Your task to perform on an android device: Open a new incognito window in Chrome Image 0: 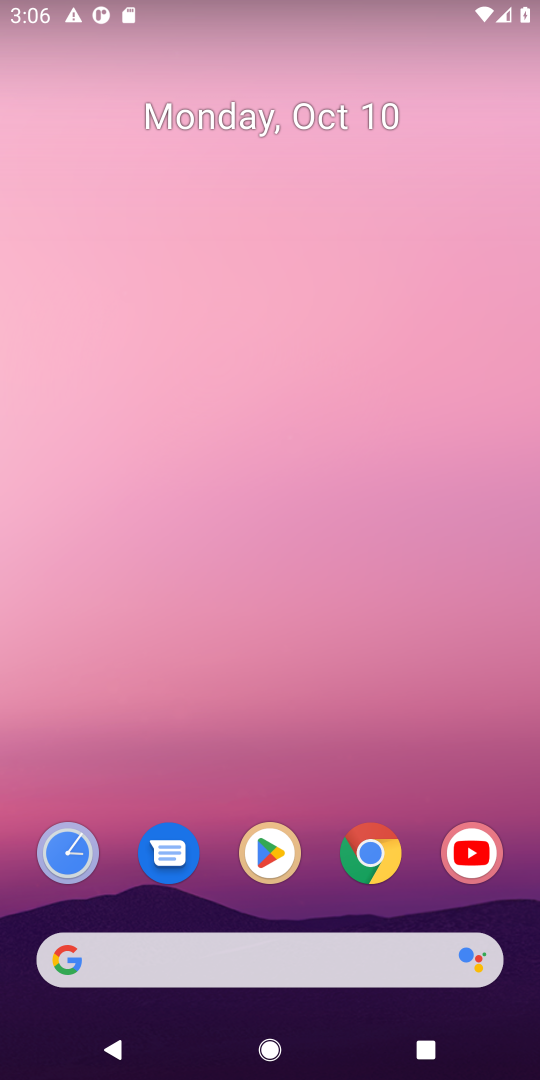
Step 0: click (369, 857)
Your task to perform on an android device: Open a new incognito window in Chrome Image 1: 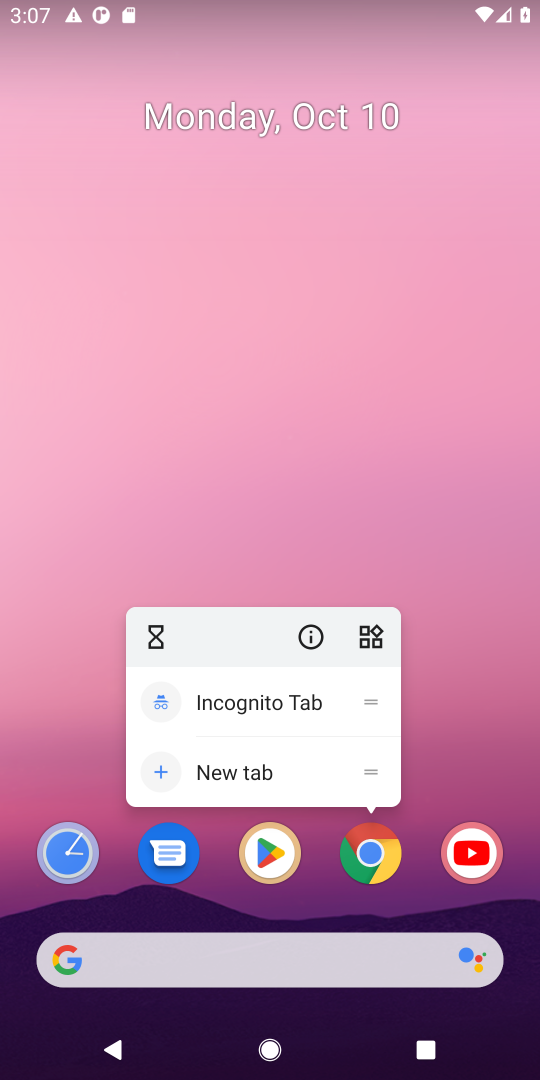
Step 1: click (357, 869)
Your task to perform on an android device: Open a new incognito window in Chrome Image 2: 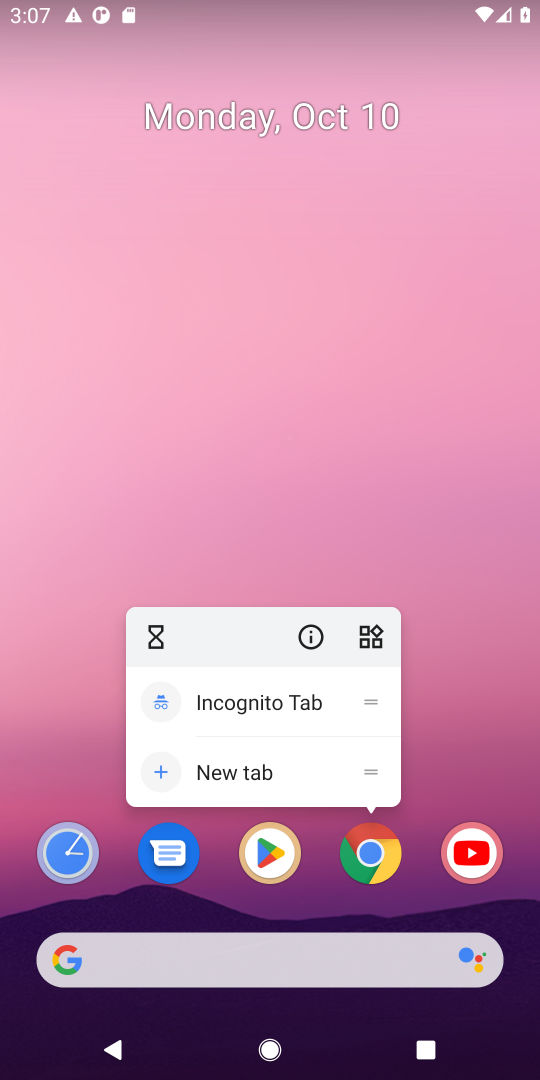
Step 2: click (396, 895)
Your task to perform on an android device: Open a new incognito window in Chrome Image 3: 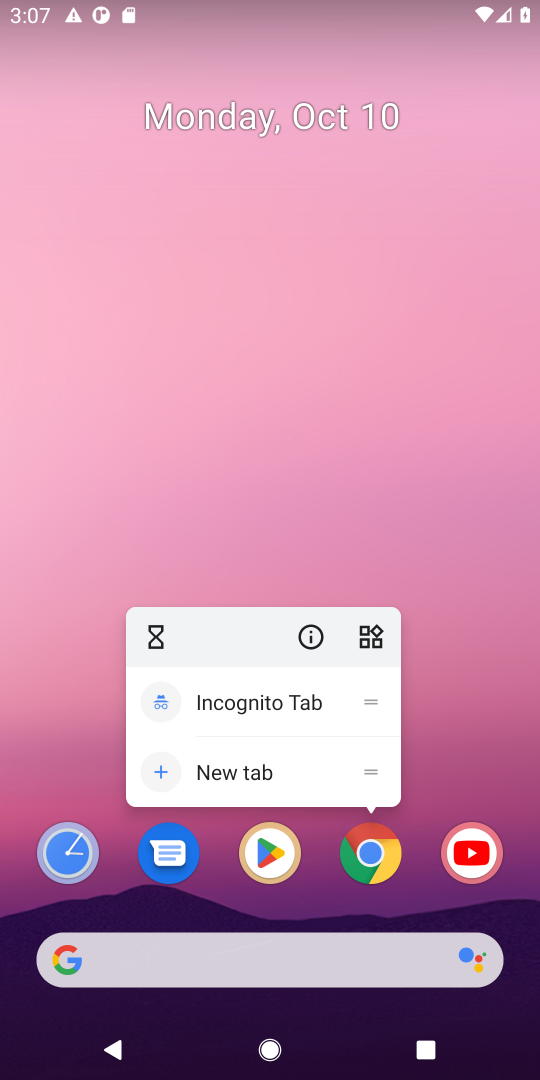
Step 3: click (301, 692)
Your task to perform on an android device: Open a new incognito window in Chrome Image 4: 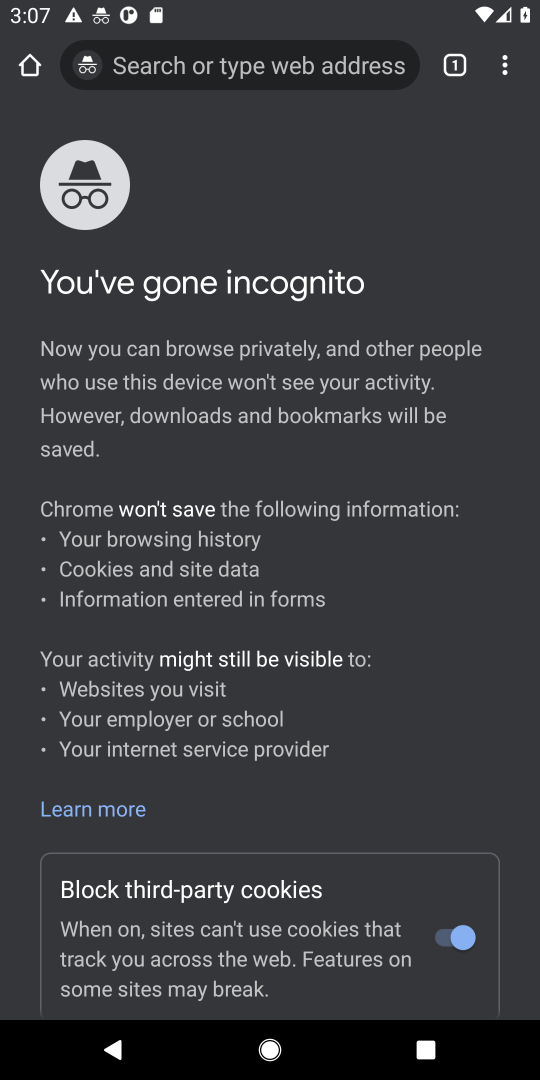
Step 4: drag from (432, 733) to (498, 186)
Your task to perform on an android device: Open a new incognito window in Chrome Image 5: 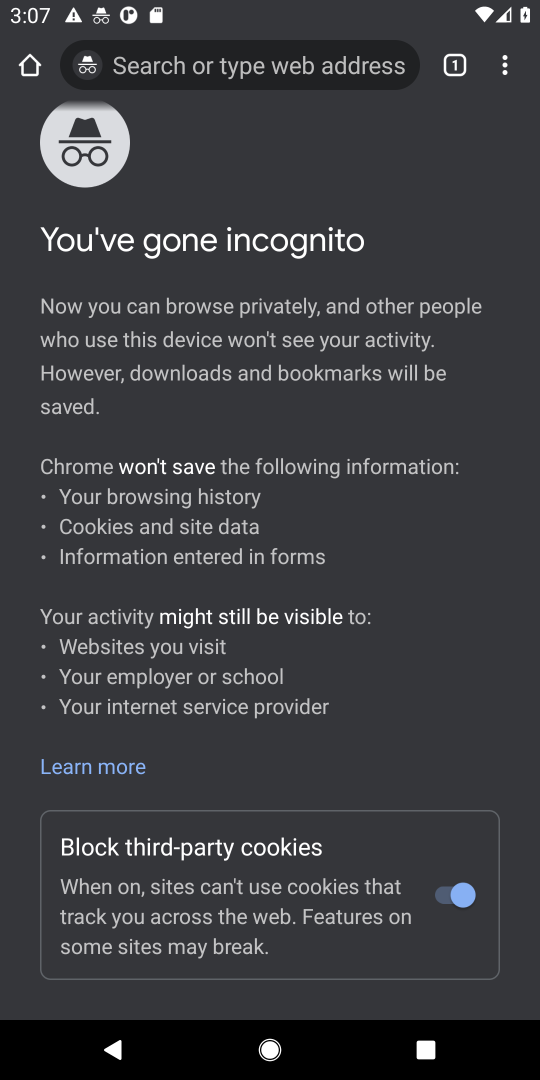
Step 5: drag from (441, 880) to (494, 305)
Your task to perform on an android device: Open a new incognito window in Chrome Image 6: 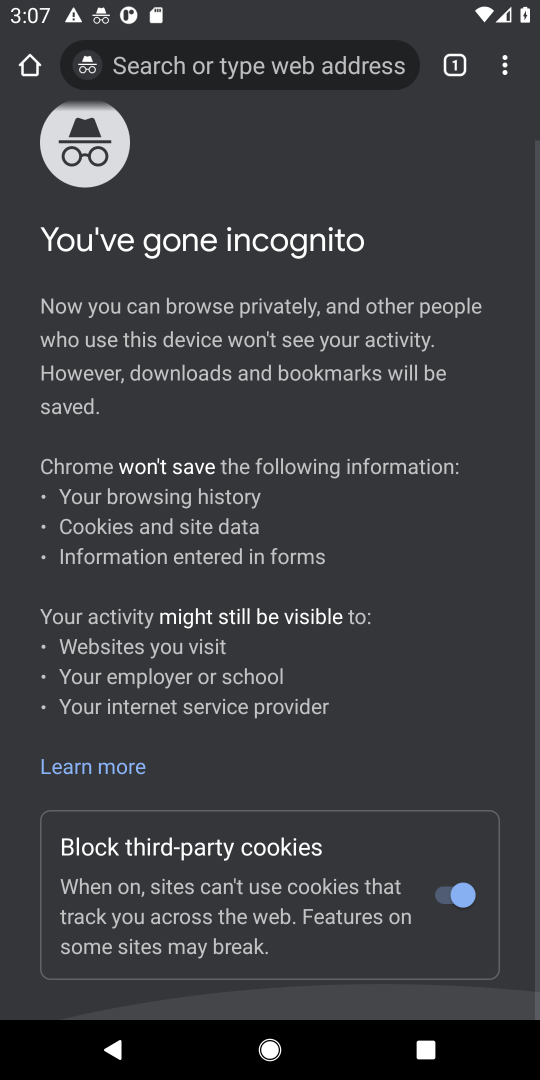
Step 6: click (131, 766)
Your task to perform on an android device: Open a new incognito window in Chrome Image 7: 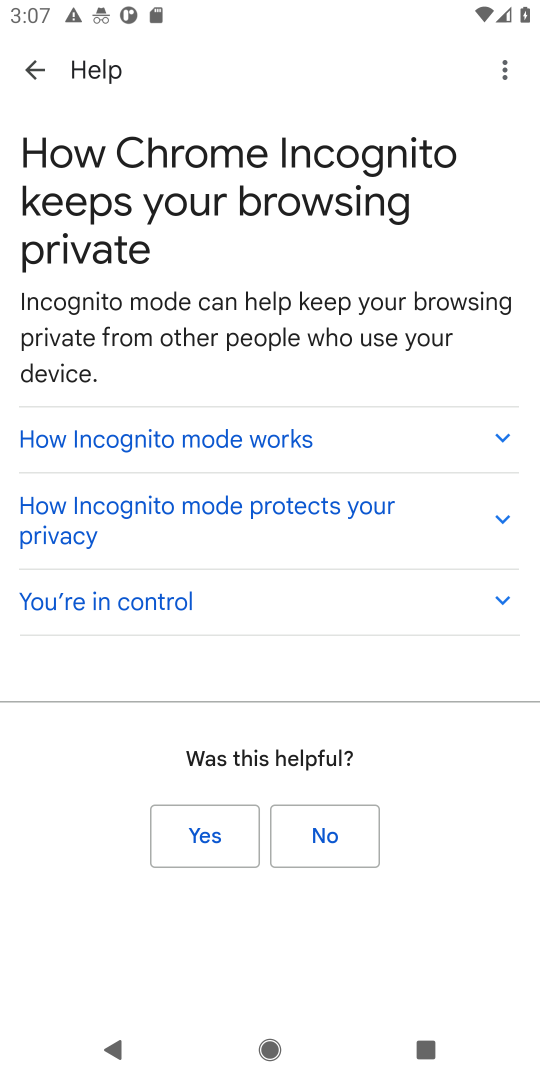
Step 7: click (348, 856)
Your task to perform on an android device: Open a new incognito window in Chrome Image 8: 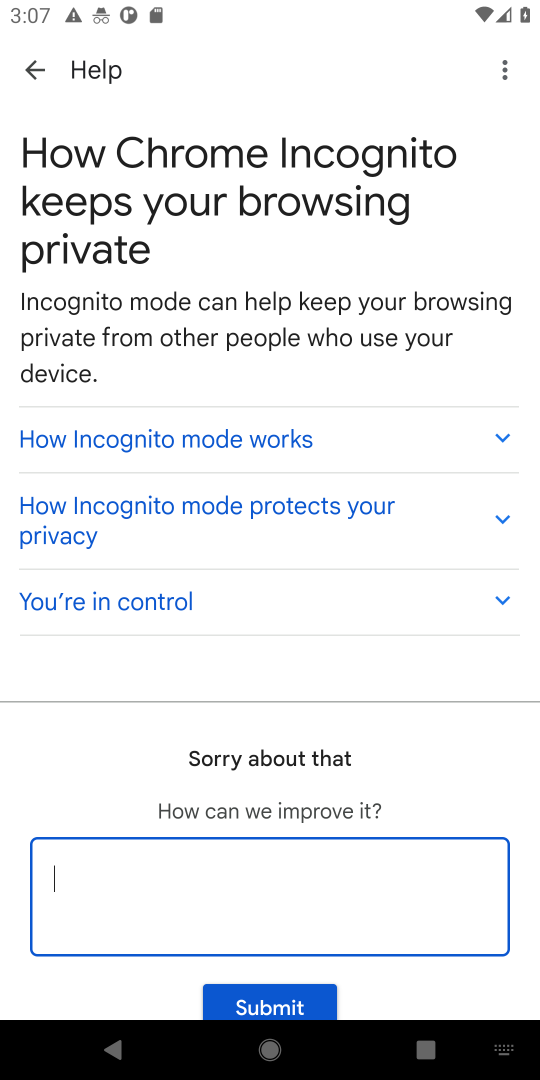
Step 8: drag from (373, 745) to (370, 140)
Your task to perform on an android device: Open a new incognito window in Chrome Image 9: 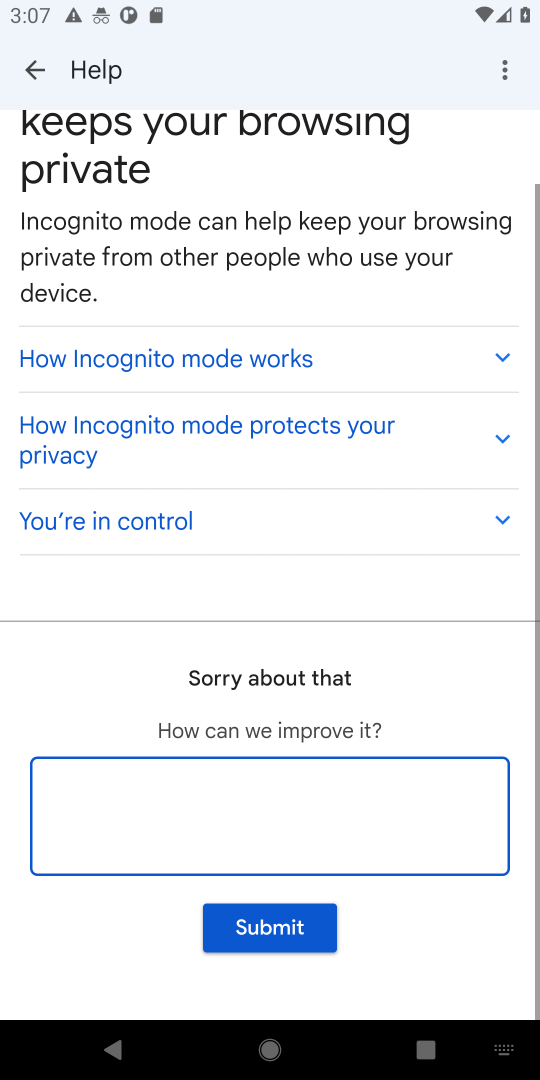
Step 9: click (28, 72)
Your task to perform on an android device: Open a new incognito window in Chrome Image 10: 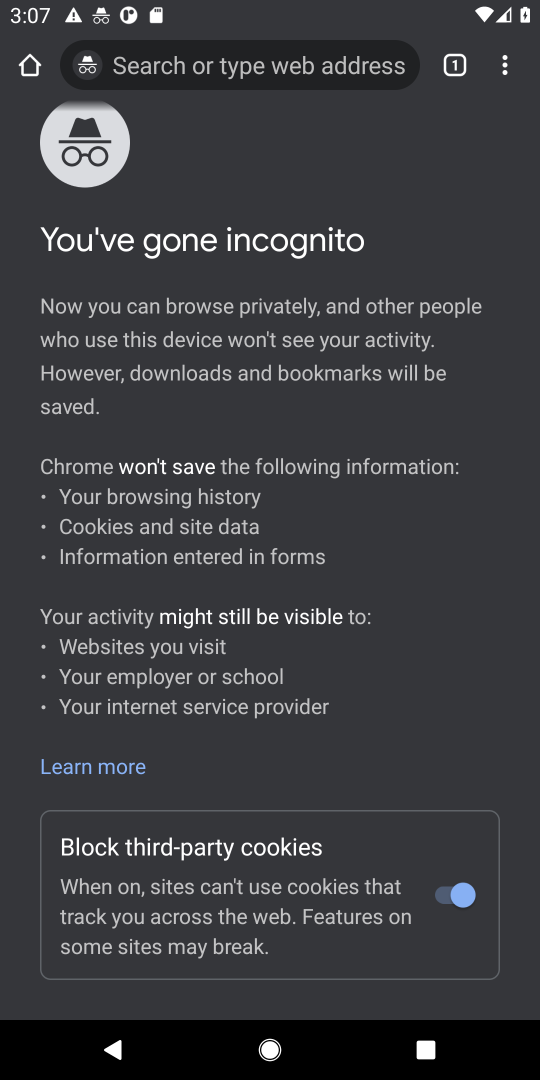
Step 10: drag from (313, 357) to (334, 130)
Your task to perform on an android device: Open a new incognito window in Chrome Image 11: 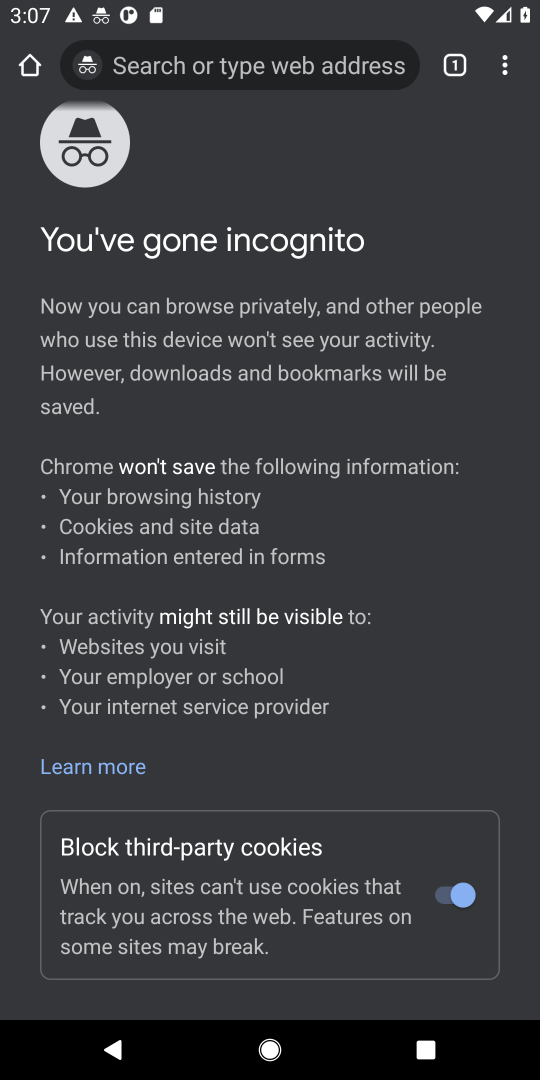
Step 11: drag from (375, 392) to (384, 241)
Your task to perform on an android device: Open a new incognito window in Chrome Image 12: 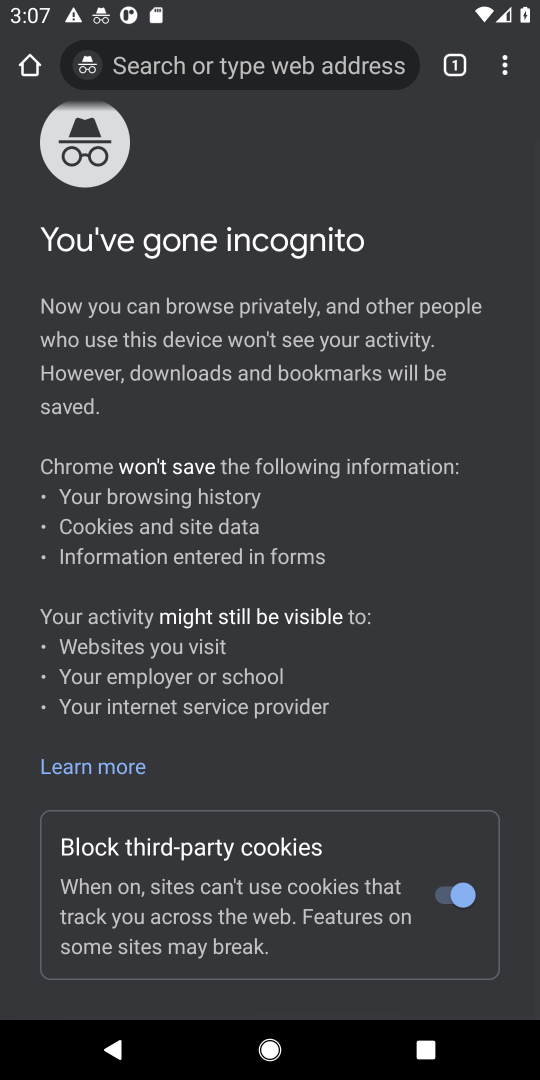
Step 12: click (212, 70)
Your task to perform on an android device: Open a new incognito window in Chrome Image 13: 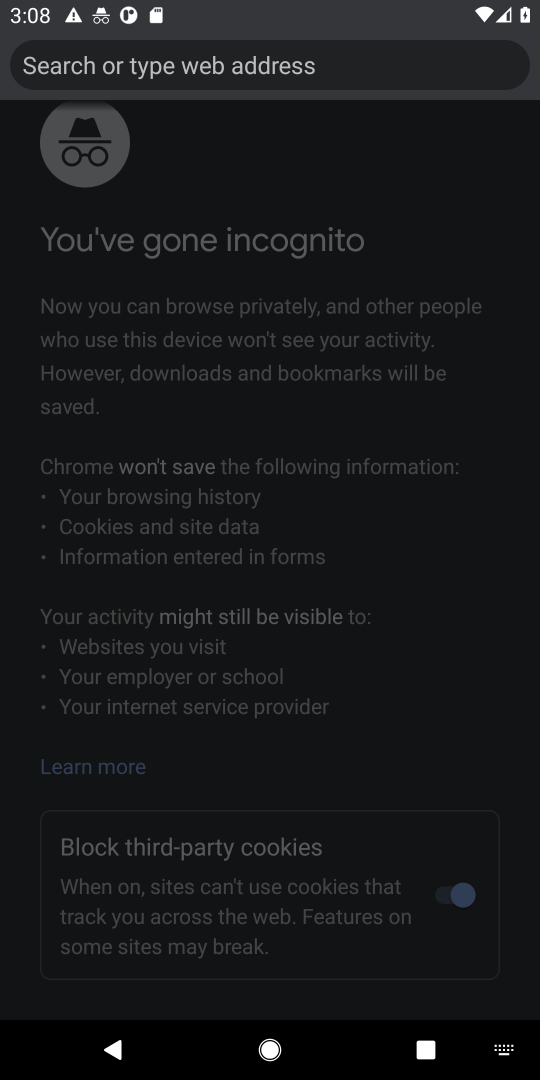
Step 13: type "cars"
Your task to perform on an android device: Open a new incognito window in Chrome Image 14: 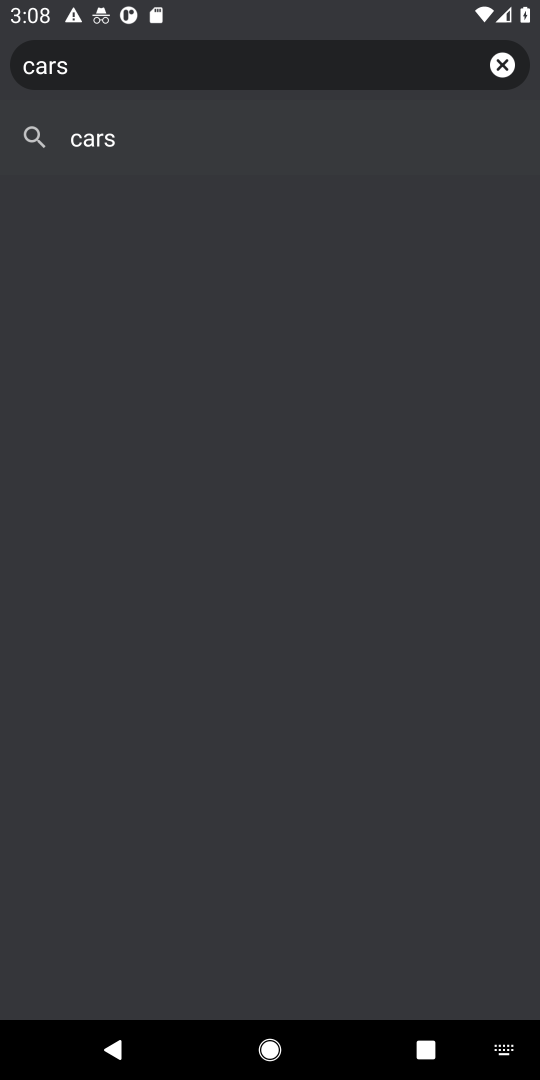
Step 14: press enter
Your task to perform on an android device: Open a new incognito window in Chrome Image 15: 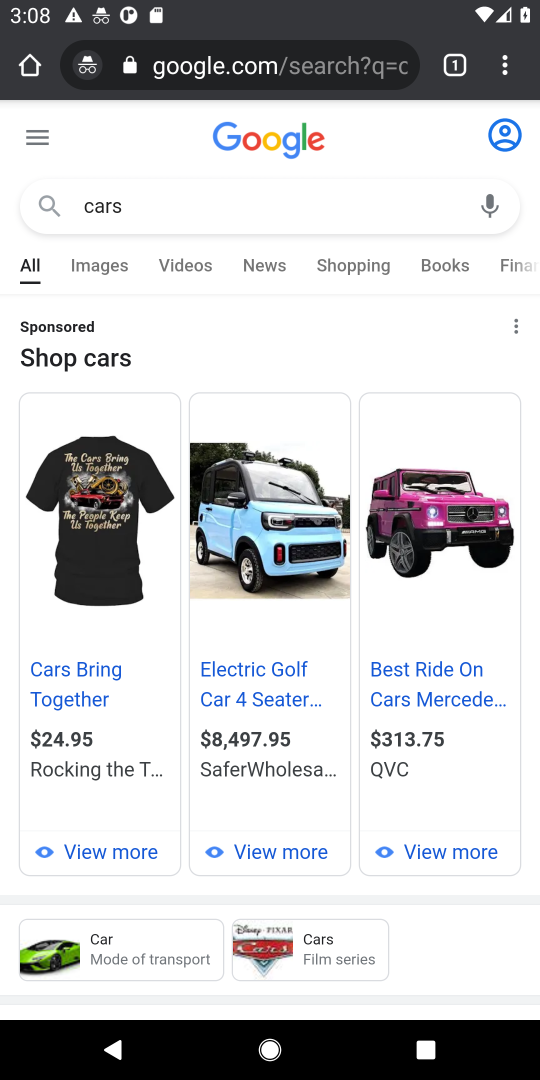
Step 15: drag from (424, 862) to (396, 96)
Your task to perform on an android device: Open a new incognito window in Chrome Image 16: 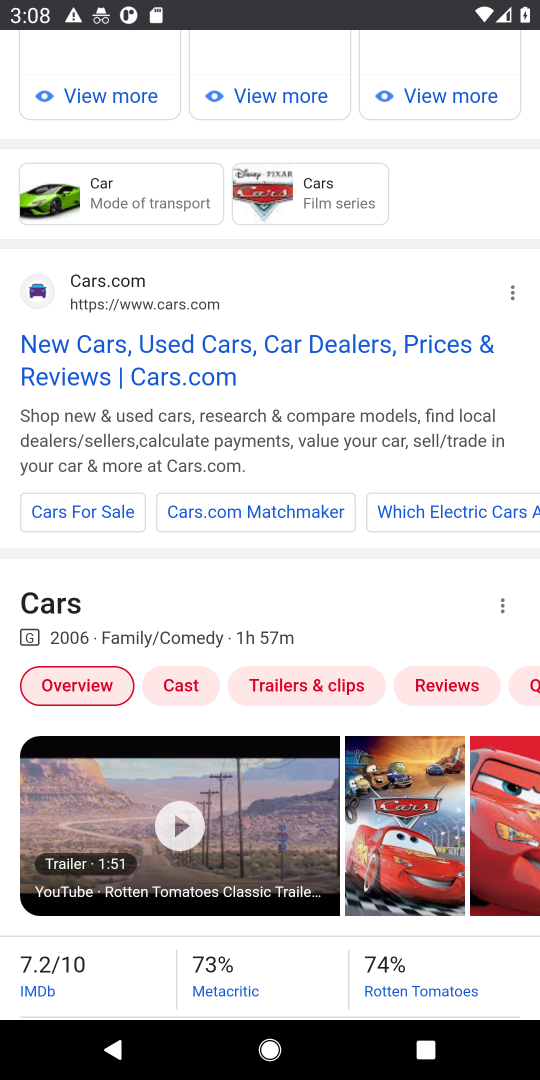
Step 16: click (242, 343)
Your task to perform on an android device: Open a new incognito window in Chrome Image 17: 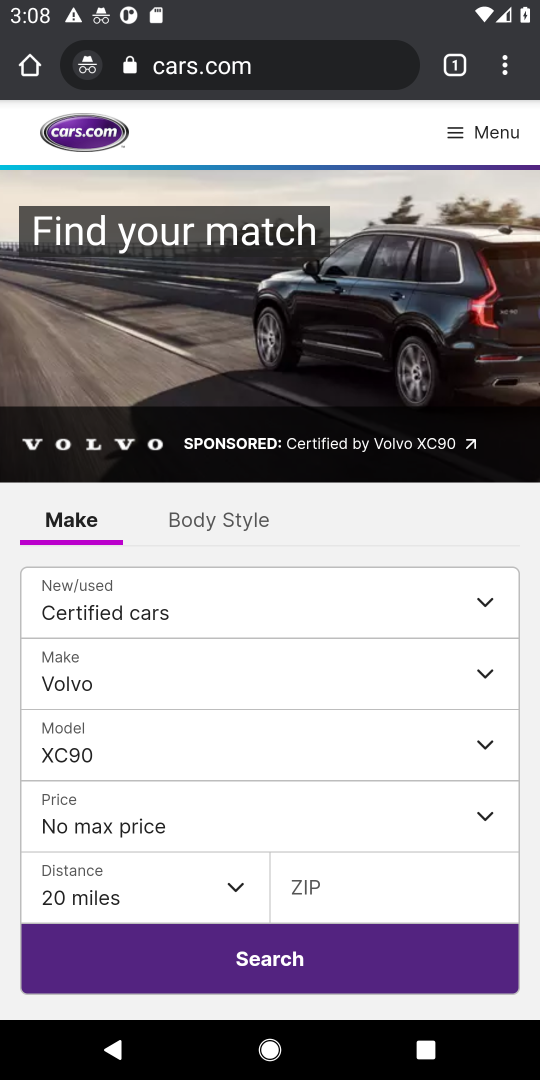
Step 17: drag from (270, 580) to (402, 117)
Your task to perform on an android device: Open a new incognito window in Chrome Image 18: 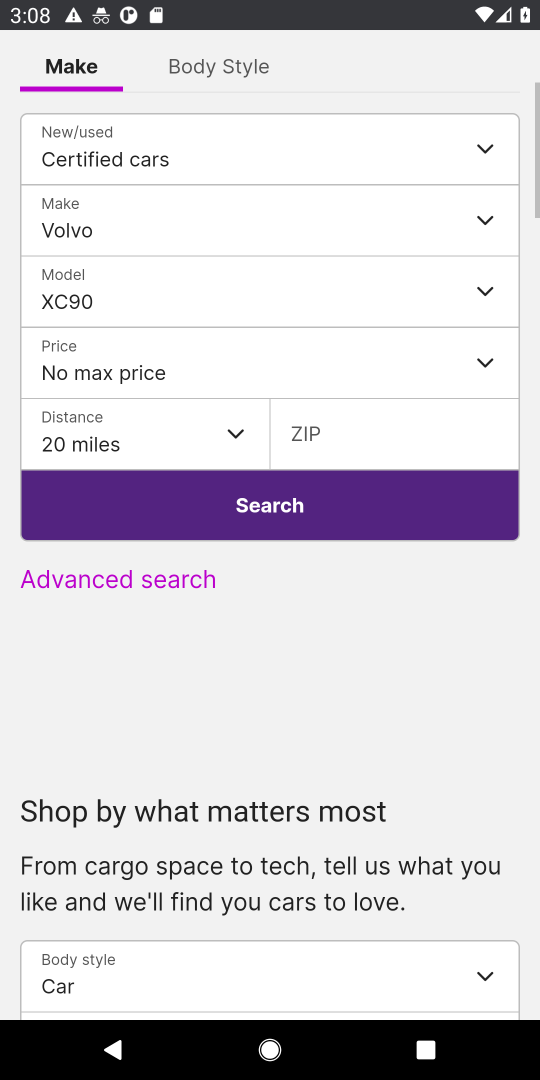
Step 18: drag from (445, 410) to (498, 110)
Your task to perform on an android device: Open a new incognito window in Chrome Image 19: 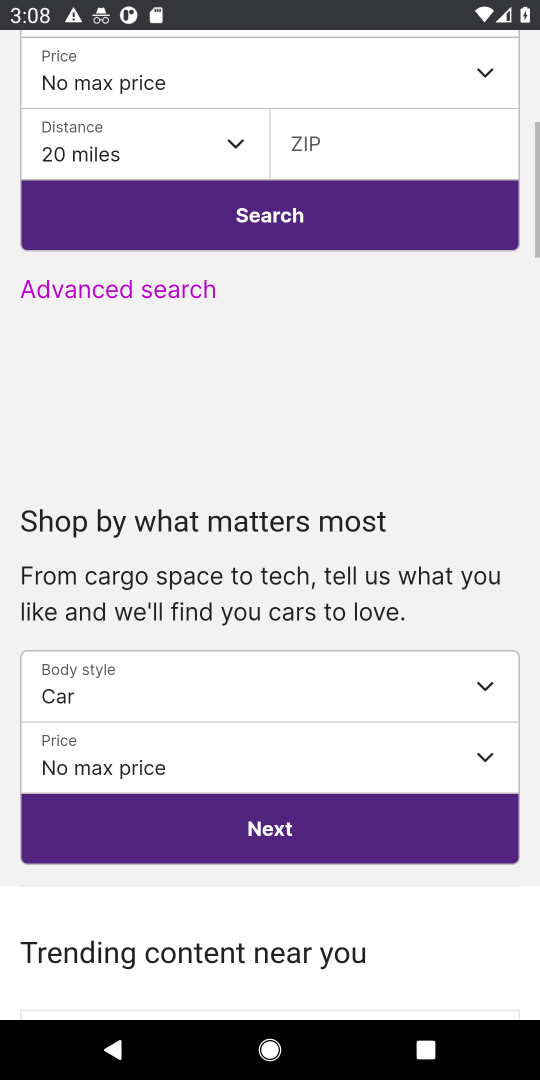
Step 19: drag from (390, 605) to (470, 225)
Your task to perform on an android device: Open a new incognito window in Chrome Image 20: 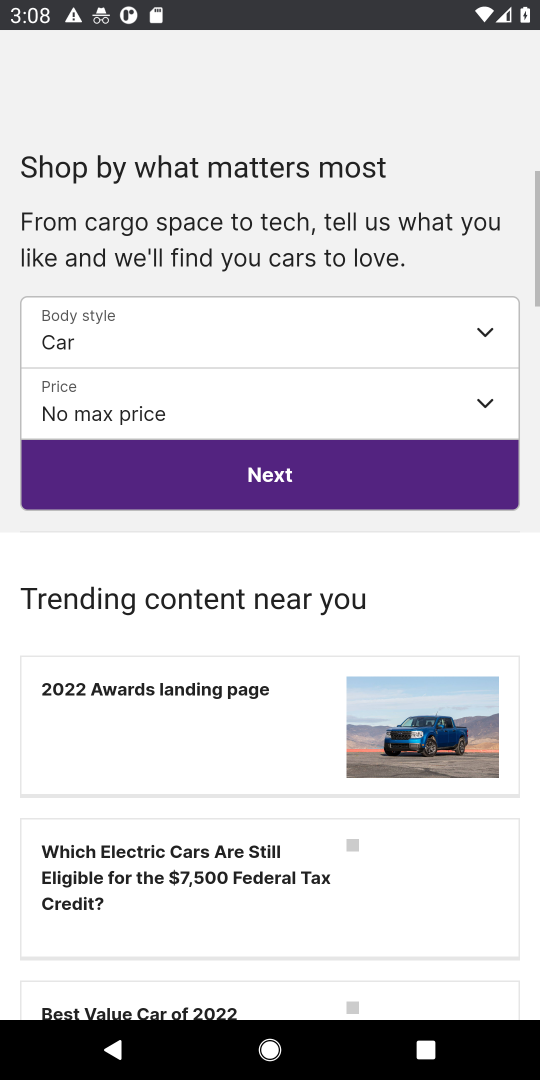
Step 20: drag from (420, 657) to (469, 151)
Your task to perform on an android device: Open a new incognito window in Chrome Image 21: 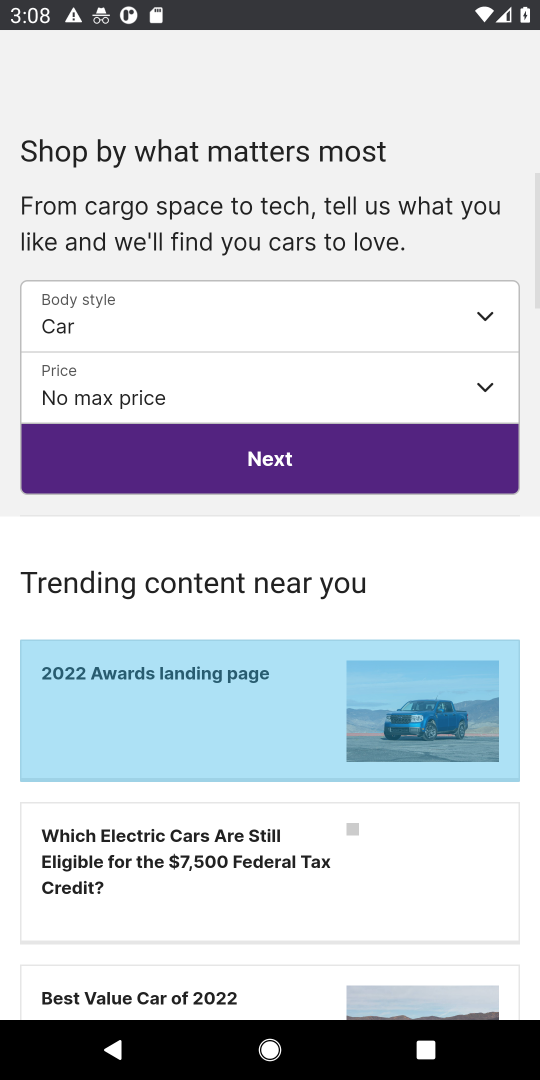
Step 21: drag from (410, 689) to (286, 243)
Your task to perform on an android device: Open a new incognito window in Chrome Image 22: 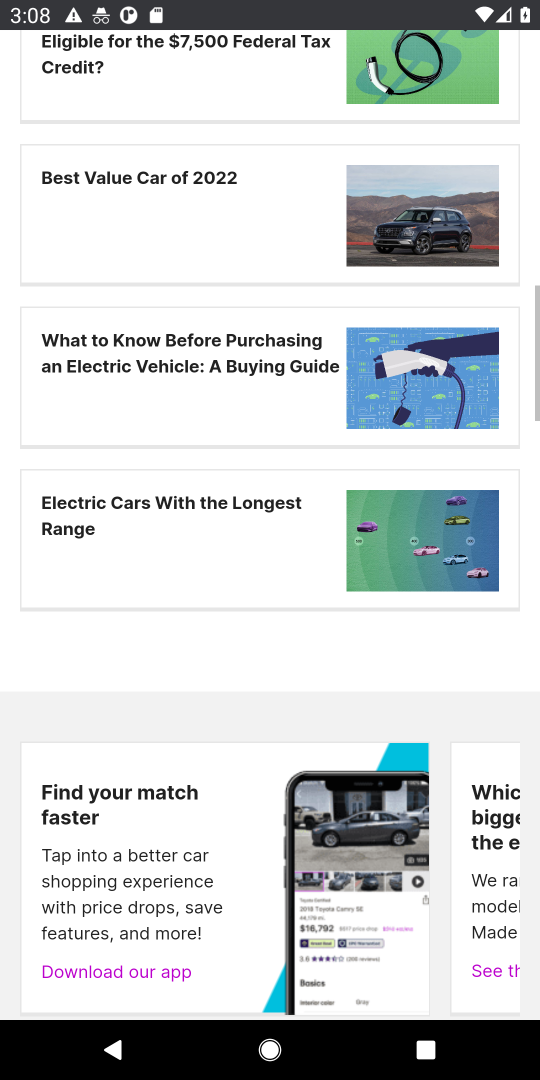
Step 22: drag from (252, 458) to (283, 200)
Your task to perform on an android device: Open a new incognito window in Chrome Image 23: 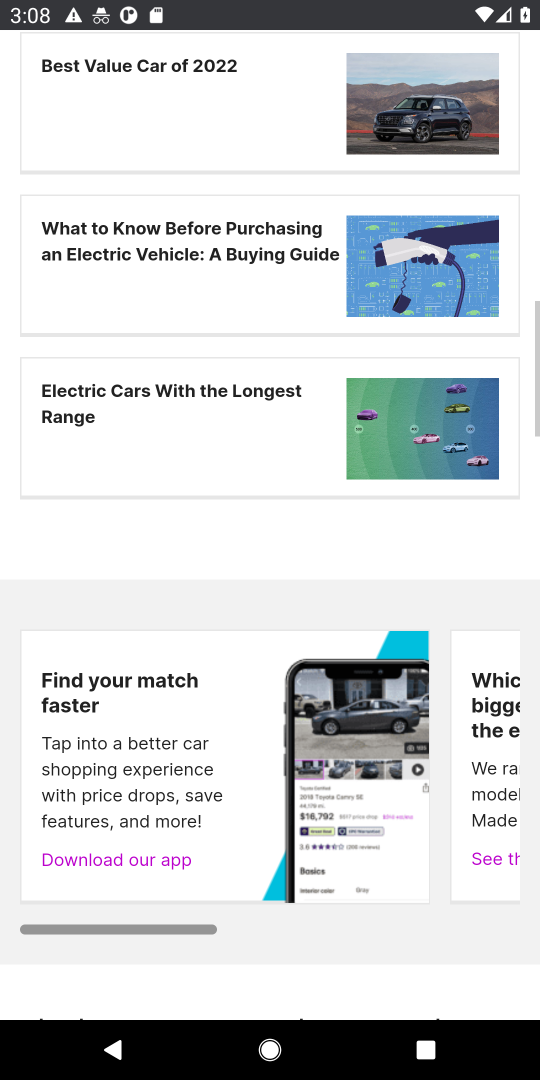
Step 23: drag from (308, 470) to (356, 265)
Your task to perform on an android device: Open a new incognito window in Chrome Image 24: 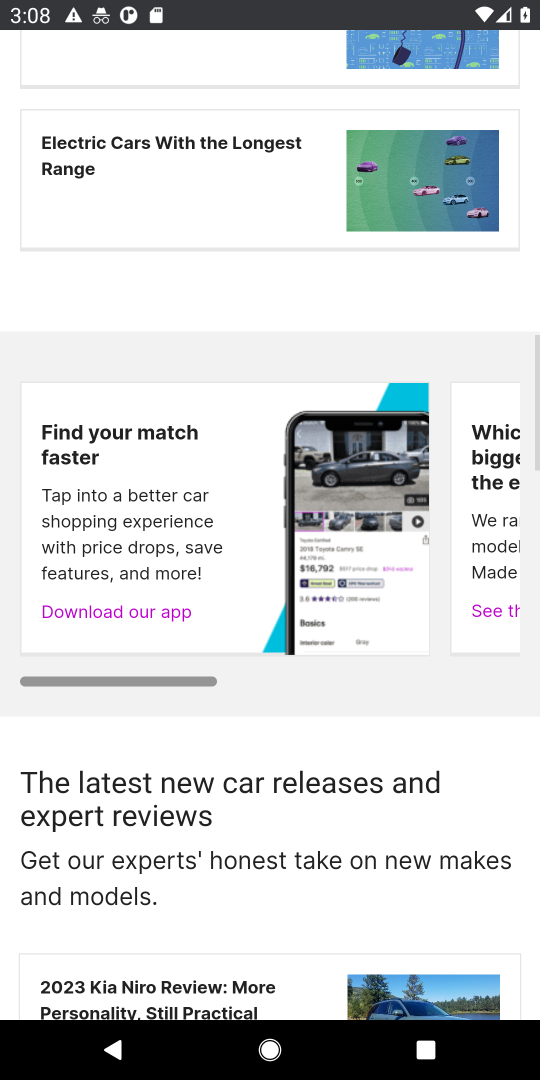
Step 24: drag from (307, 668) to (357, 192)
Your task to perform on an android device: Open a new incognito window in Chrome Image 25: 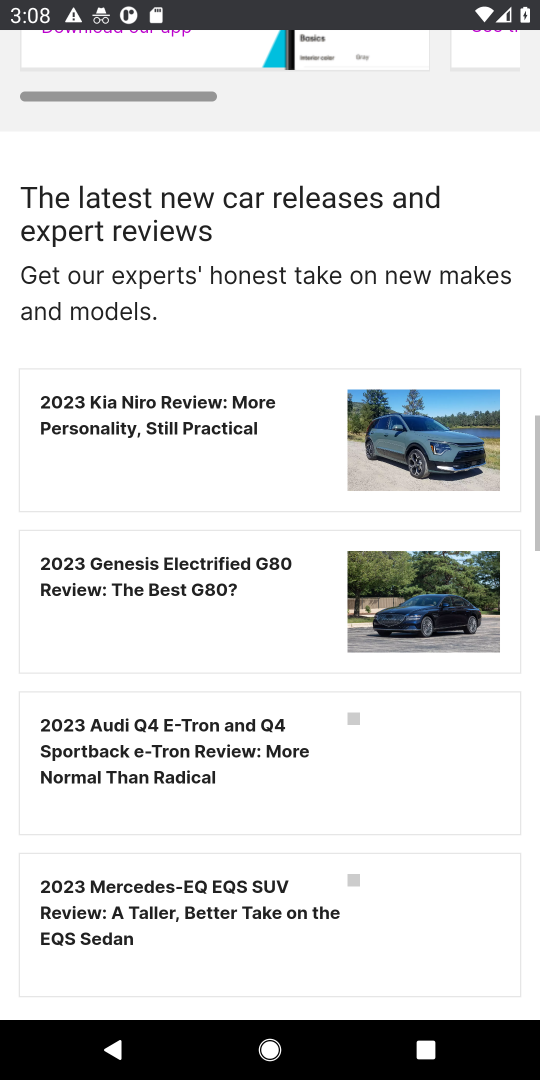
Step 25: drag from (375, 337) to (385, 184)
Your task to perform on an android device: Open a new incognito window in Chrome Image 26: 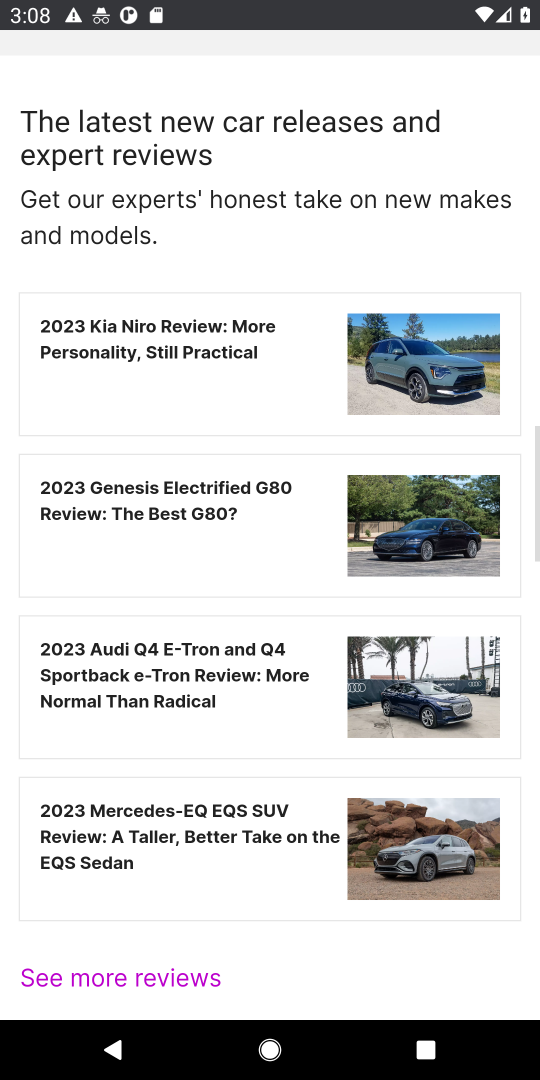
Step 26: drag from (324, 525) to (381, 121)
Your task to perform on an android device: Open a new incognito window in Chrome Image 27: 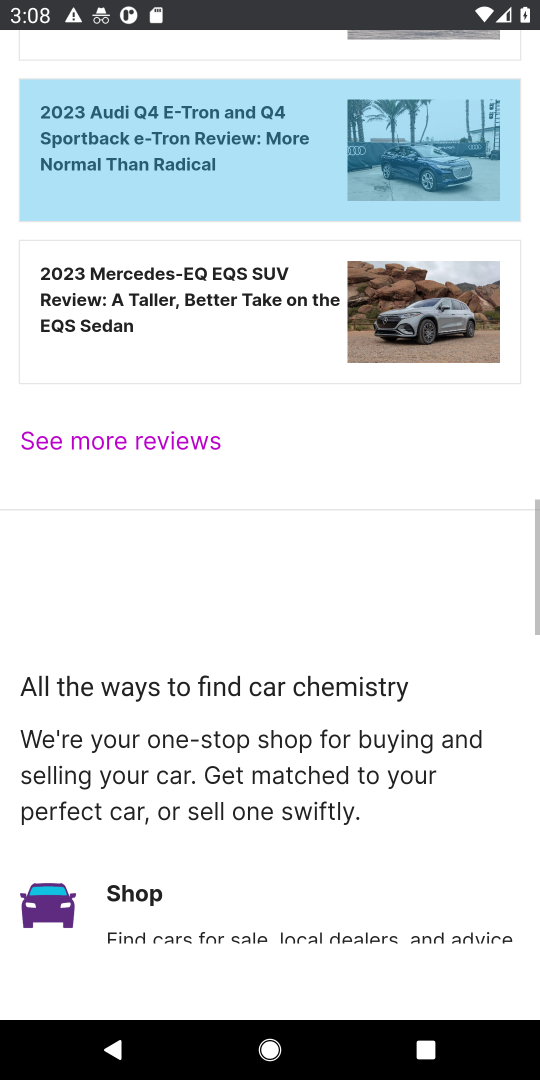
Step 27: drag from (281, 705) to (334, 93)
Your task to perform on an android device: Open a new incognito window in Chrome Image 28: 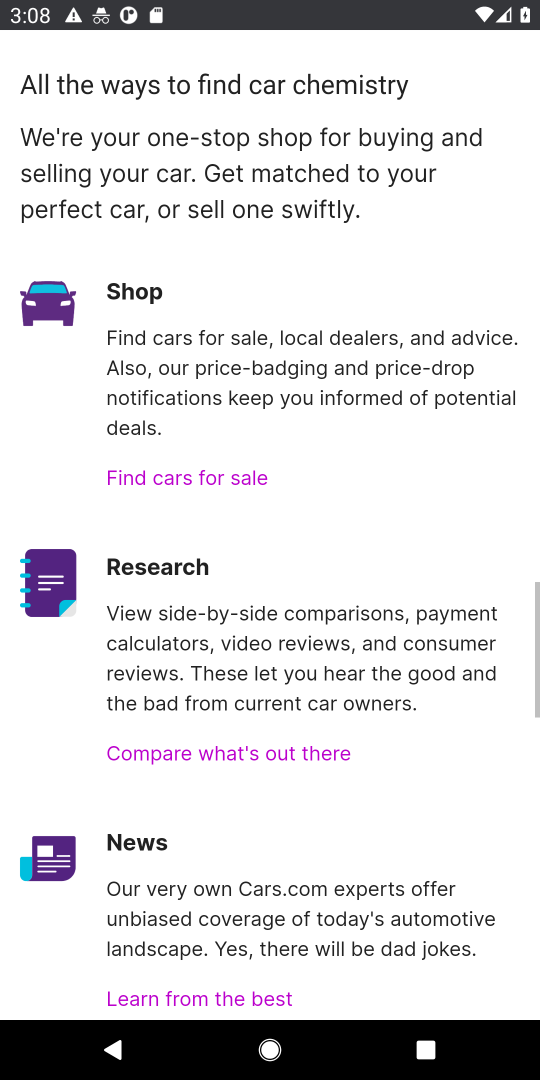
Step 28: drag from (332, 619) to (379, 121)
Your task to perform on an android device: Open a new incognito window in Chrome Image 29: 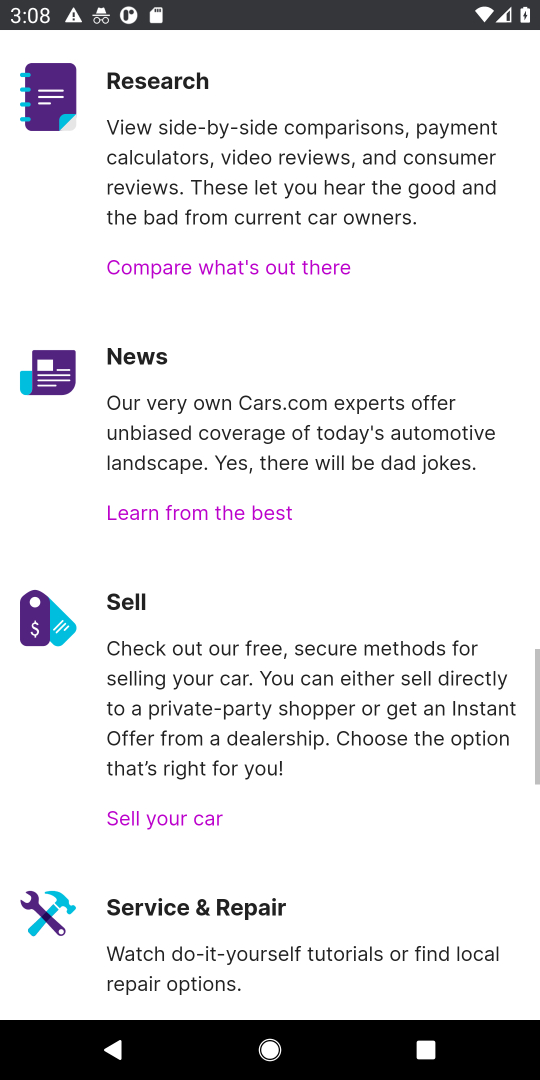
Step 29: drag from (360, 737) to (453, 289)
Your task to perform on an android device: Open a new incognito window in Chrome Image 30: 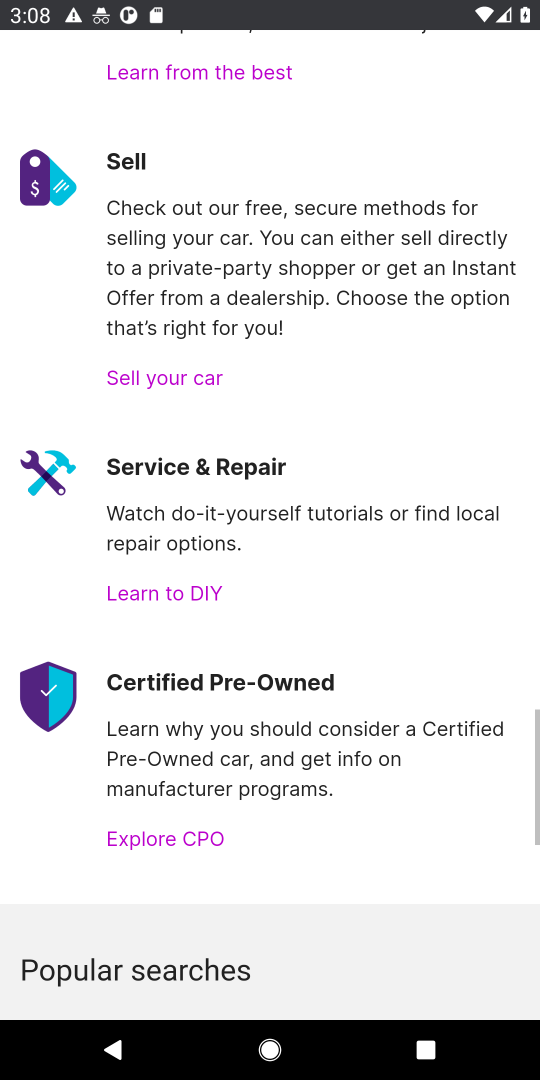
Step 30: drag from (405, 786) to (456, 396)
Your task to perform on an android device: Open a new incognito window in Chrome Image 31: 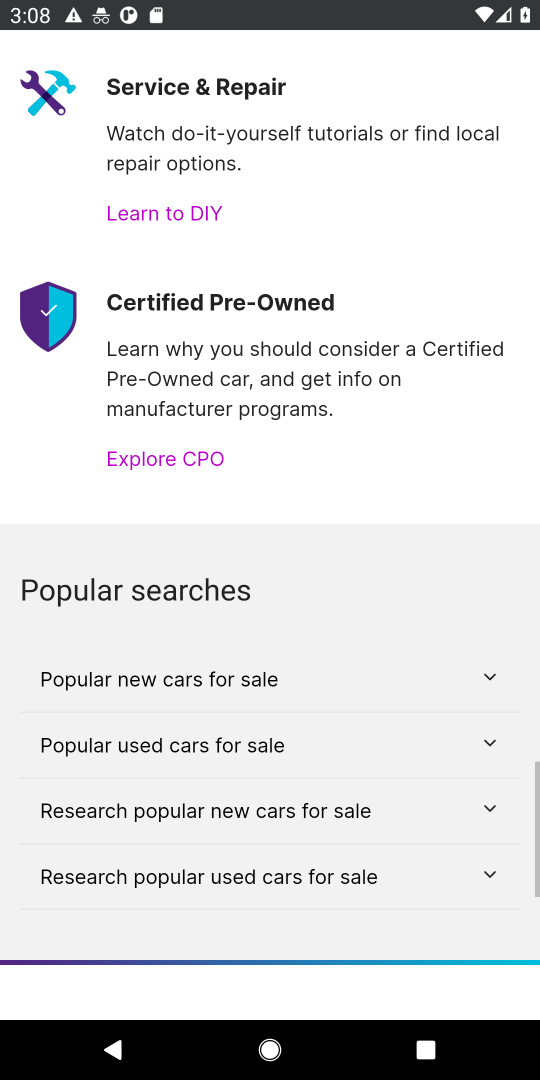
Step 31: drag from (464, 762) to (493, 609)
Your task to perform on an android device: Open a new incognito window in Chrome Image 32: 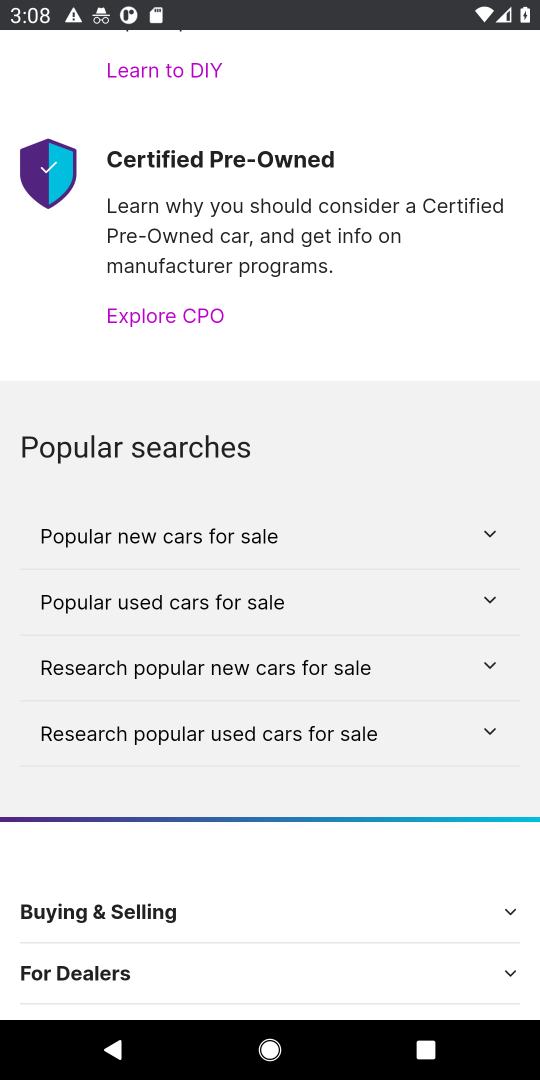
Step 32: drag from (506, 800) to (530, 376)
Your task to perform on an android device: Open a new incognito window in Chrome Image 33: 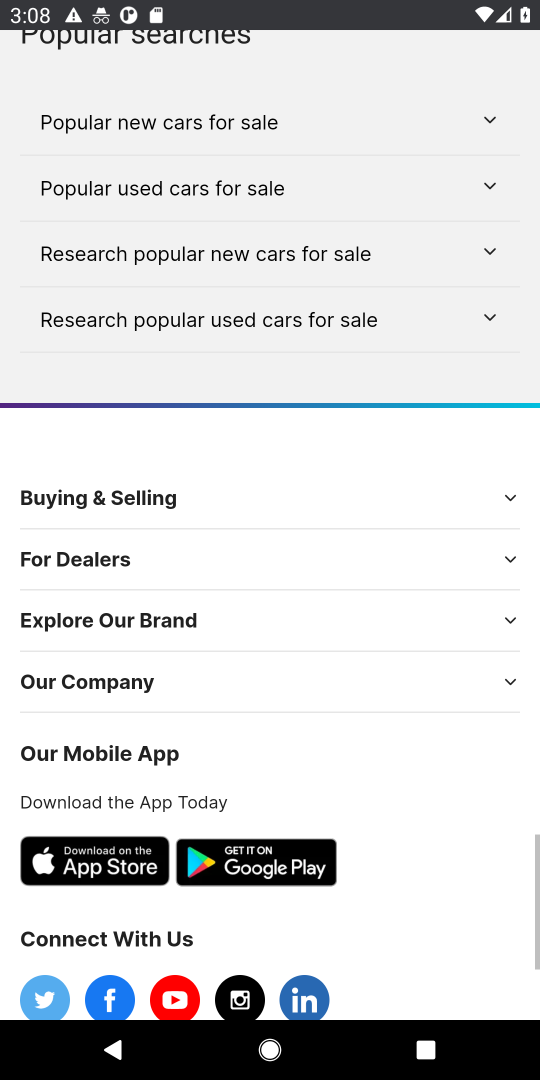
Step 33: drag from (504, 776) to (481, 451)
Your task to perform on an android device: Open a new incognito window in Chrome Image 34: 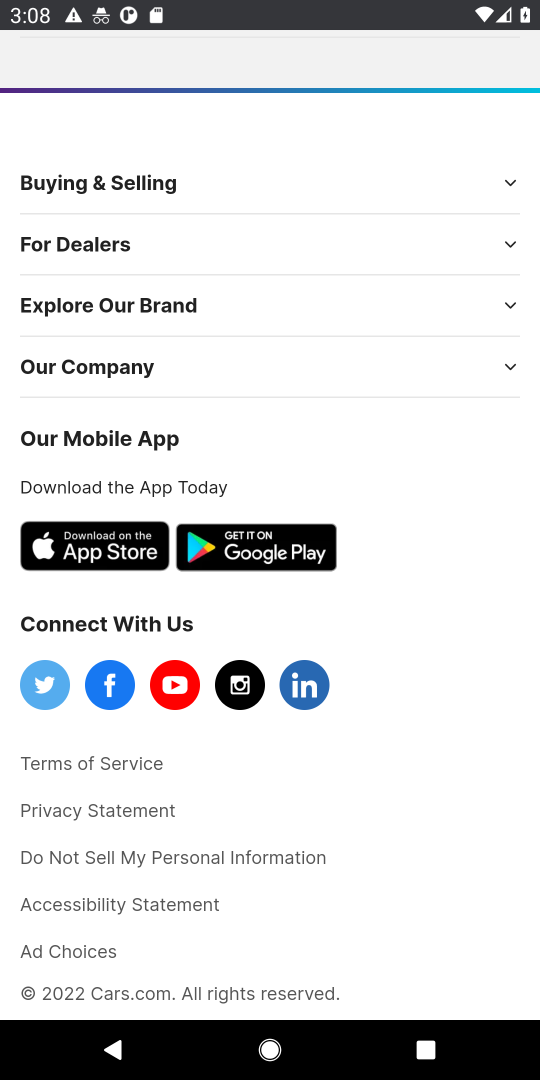
Step 34: drag from (442, 631) to (449, 445)
Your task to perform on an android device: Open a new incognito window in Chrome Image 35: 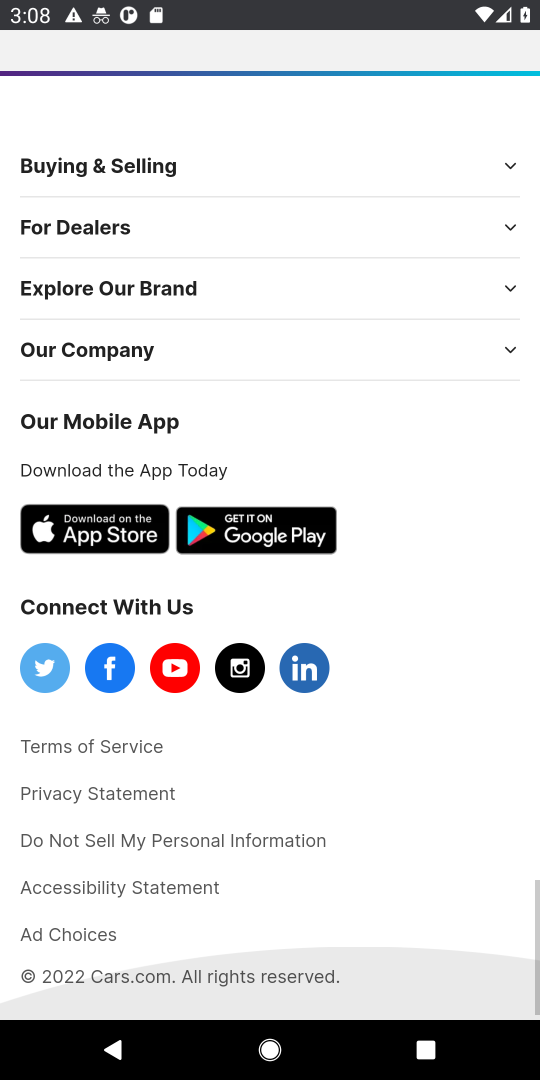
Step 35: drag from (410, 624) to (433, 442)
Your task to perform on an android device: Open a new incognito window in Chrome Image 36: 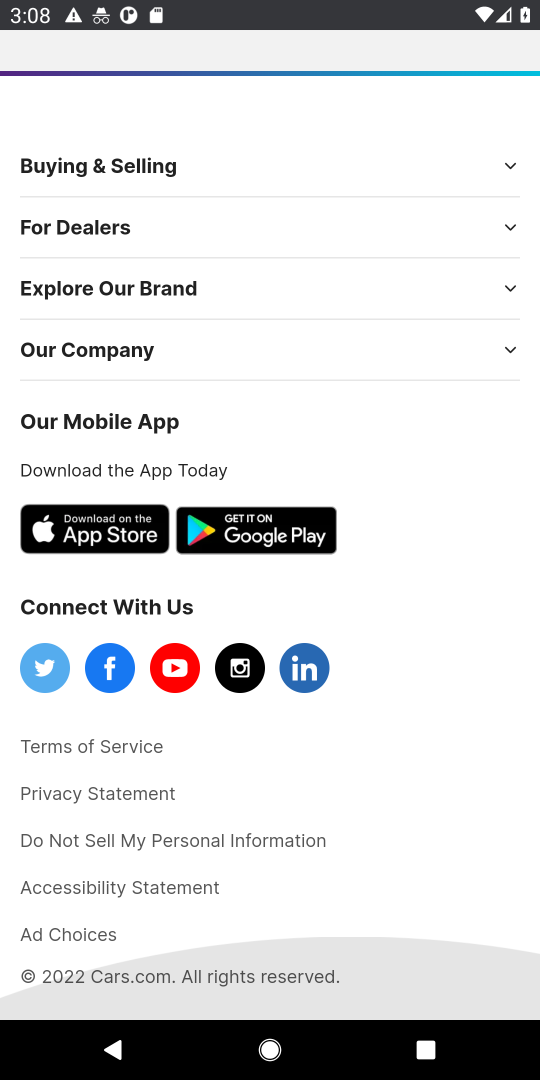
Step 36: drag from (400, 640) to (440, 388)
Your task to perform on an android device: Open a new incognito window in Chrome Image 37: 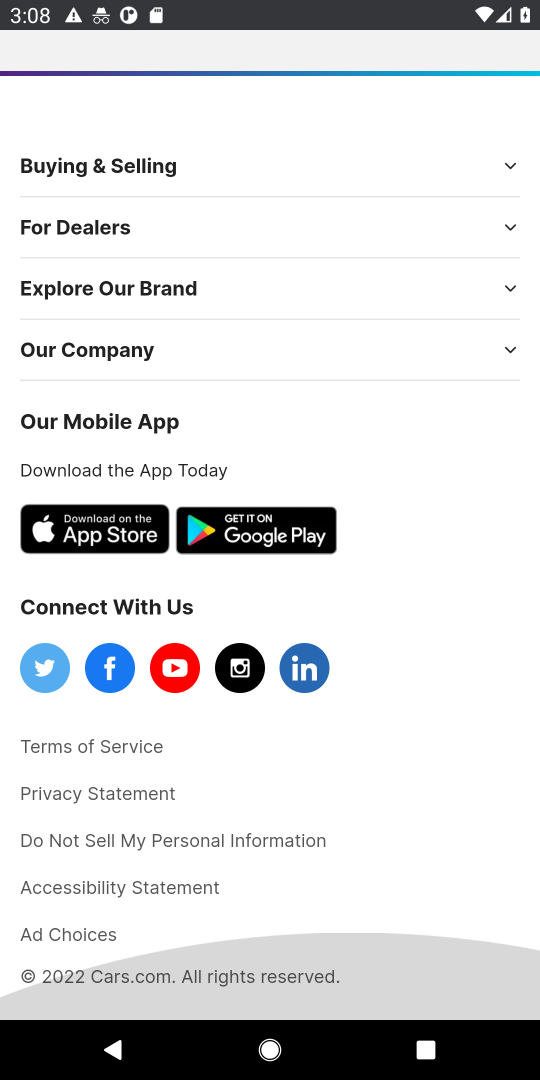
Step 37: drag from (444, 642) to (435, 296)
Your task to perform on an android device: Open a new incognito window in Chrome Image 38: 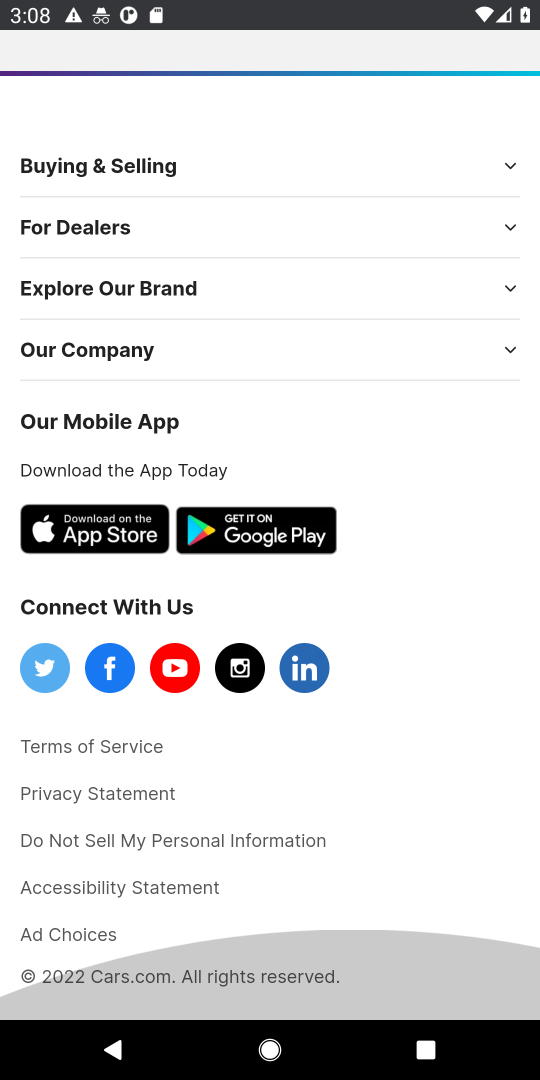
Step 38: drag from (448, 253) to (442, 778)
Your task to perform on an android device: Open a new incognito window in Chrome Image 39: 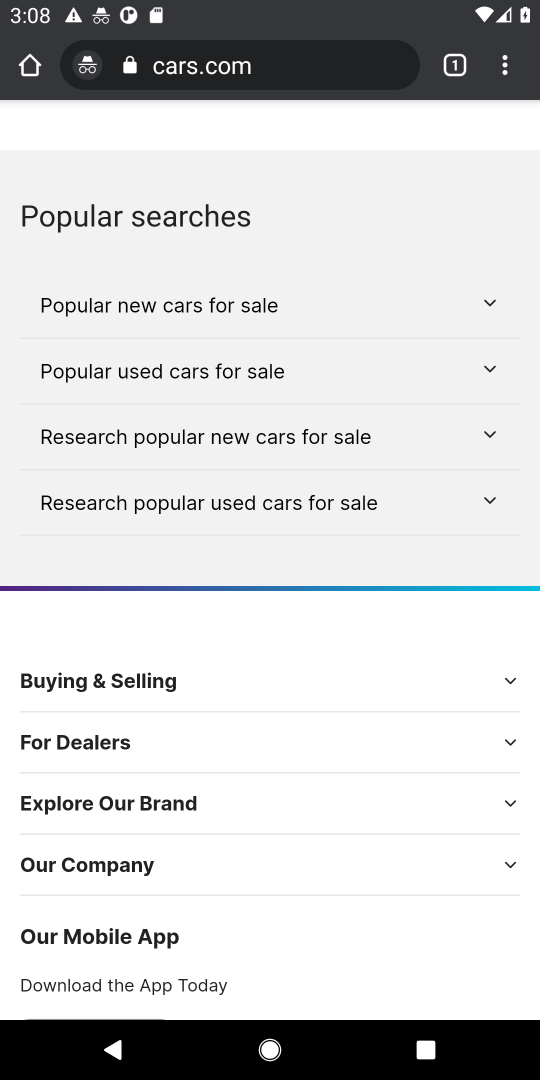
Step 39: press back button
Your task to perform on an android device: Open a new incognito window in Chrome Image 40: 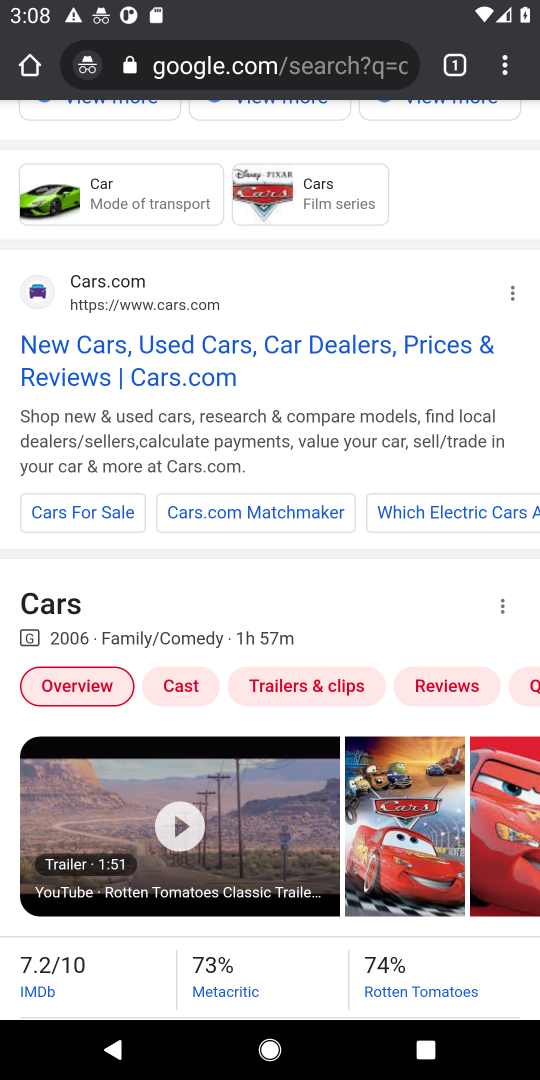
Step 40: drag from (337, 473) to (382, 112)
Your task to perform on an android device: Open a new incognito window in Chrome Image 41: 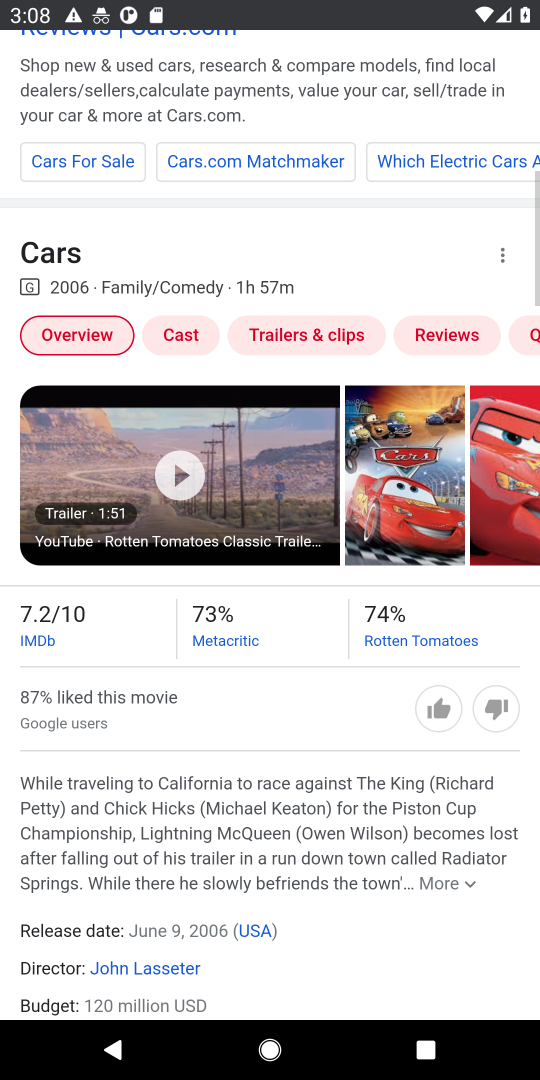
Step 41: drag from (364, 759) to (419, 158)
Your task to perform on an android device: Open a new incognito window in Chrome Image 42: 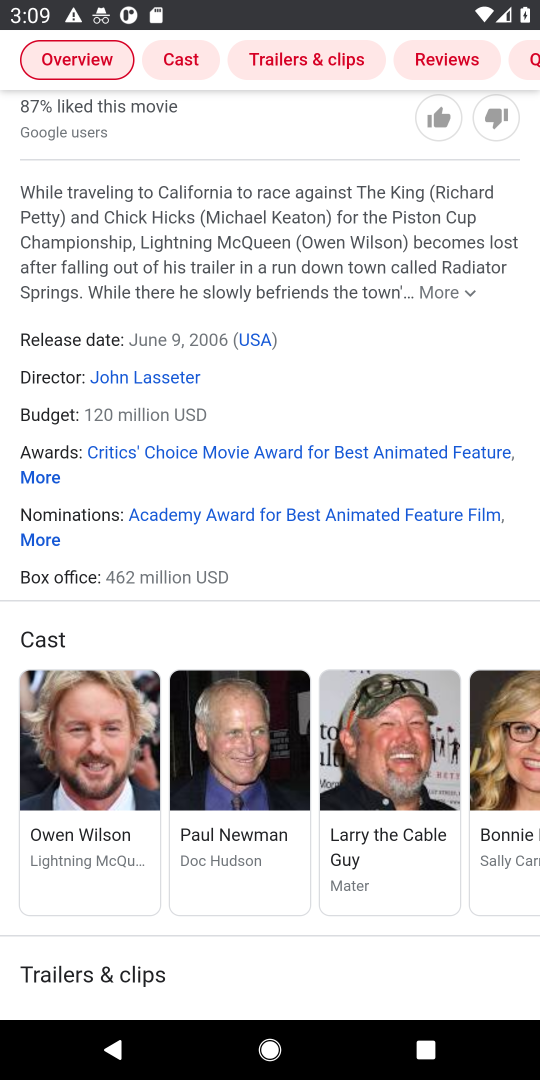
Step 42: drag from (292, 807) to (338, 190)
Your task to perform on an android device: Open a new incognito window in Chrome Image 43: 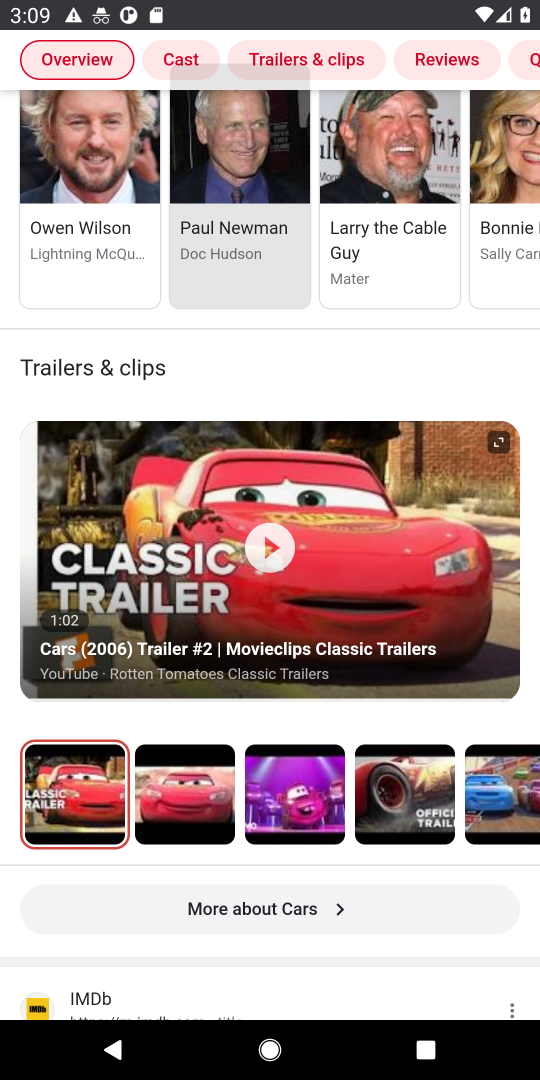
Step 43: drag from (301, 888) to (362, 165)
Your task to perform on an android device: Open a new incognito window in Chrome Image 44: 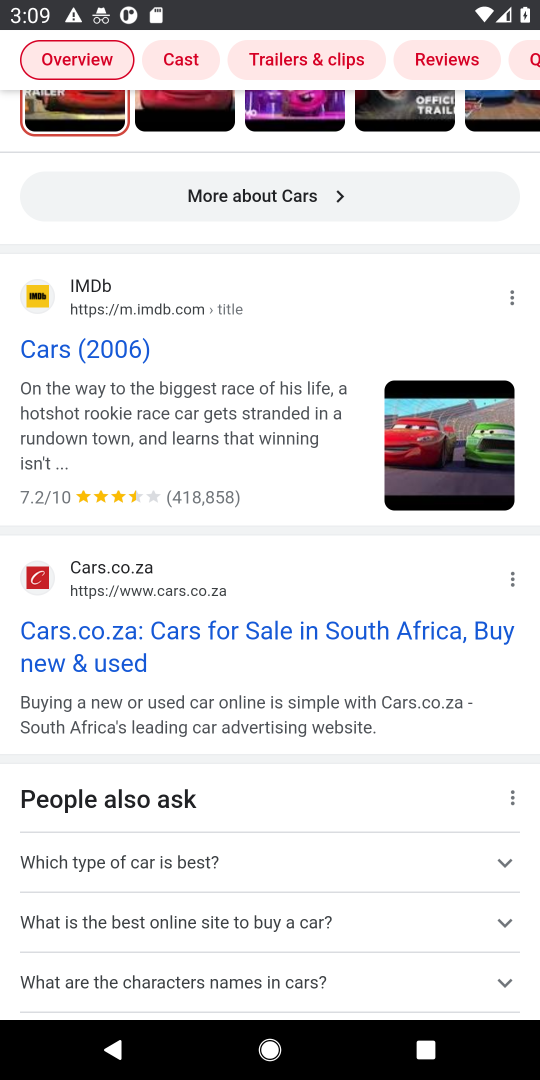
Step 44: click (107, 361)
Your task to perform on an android device: Open a new incognito window in Chrome Image 45: 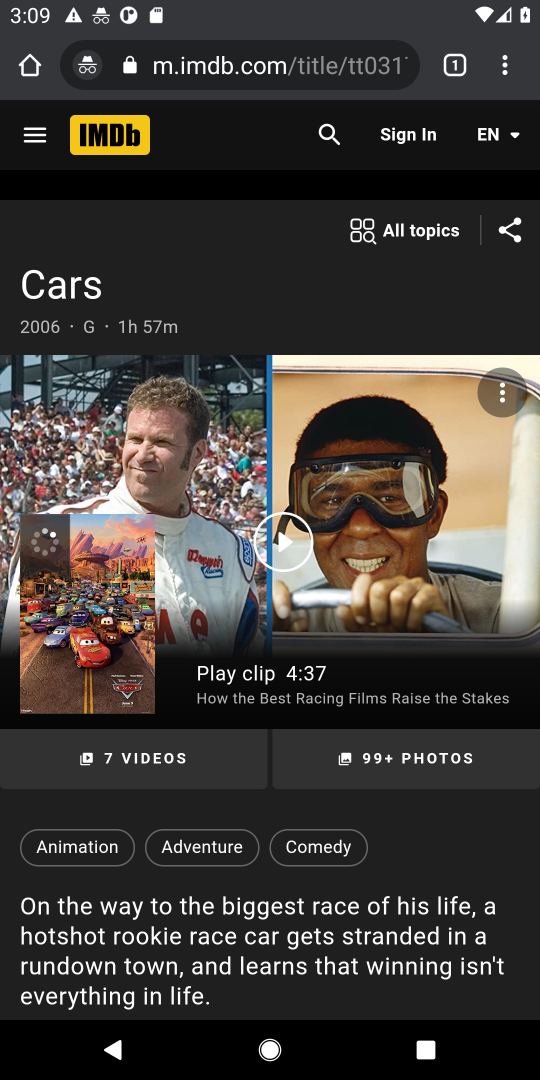
Step 45: drag from (287, 457) to (306, 268)
Your task to perform on an android device: Open a new incognito window in Chrome Image 46: 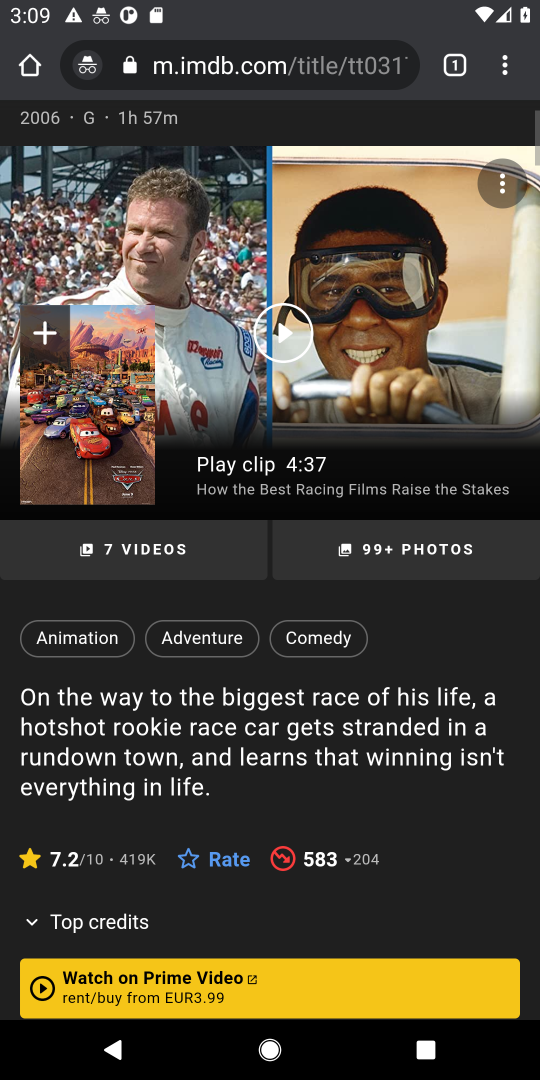
Step 46: drag from (344, 657) to (360, 328)
Your task to perform on an android device: Open a new incognito window in Chrome Image 47: 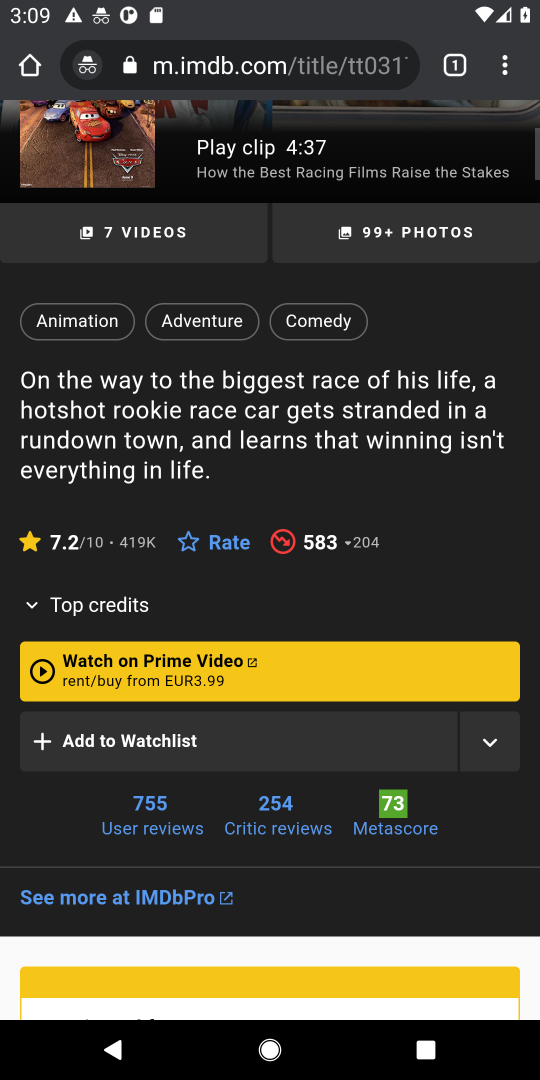
Step 47: drag from (384, 523) to (422, 288)
Your task to perform on an android device: Open a new incognito window in Chrome Image 48: 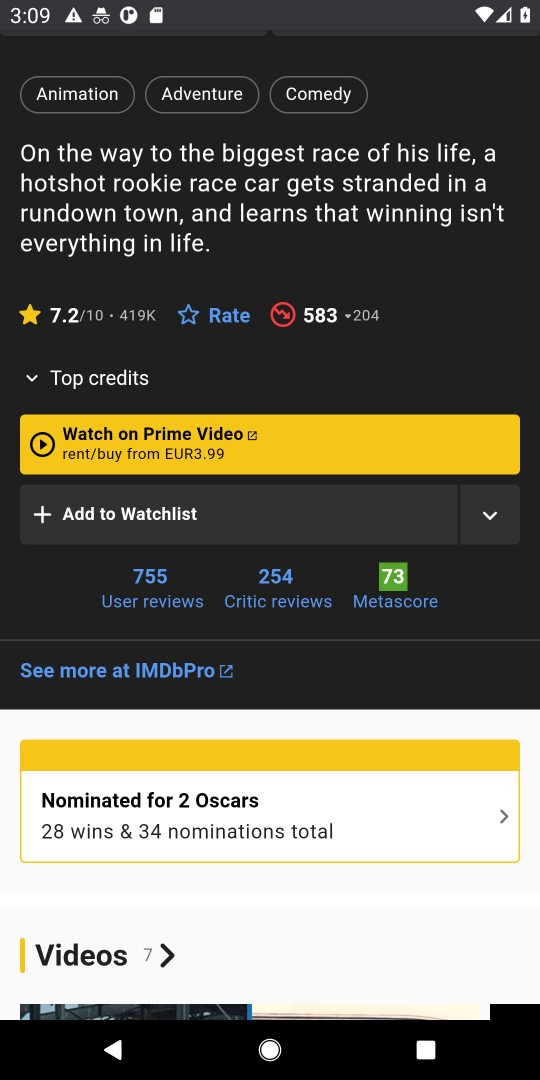
Step 48: drag from (403, 705) to (444, 395)
Your task to perform on an android device: Open a new incognito window in Chrome Image 49: 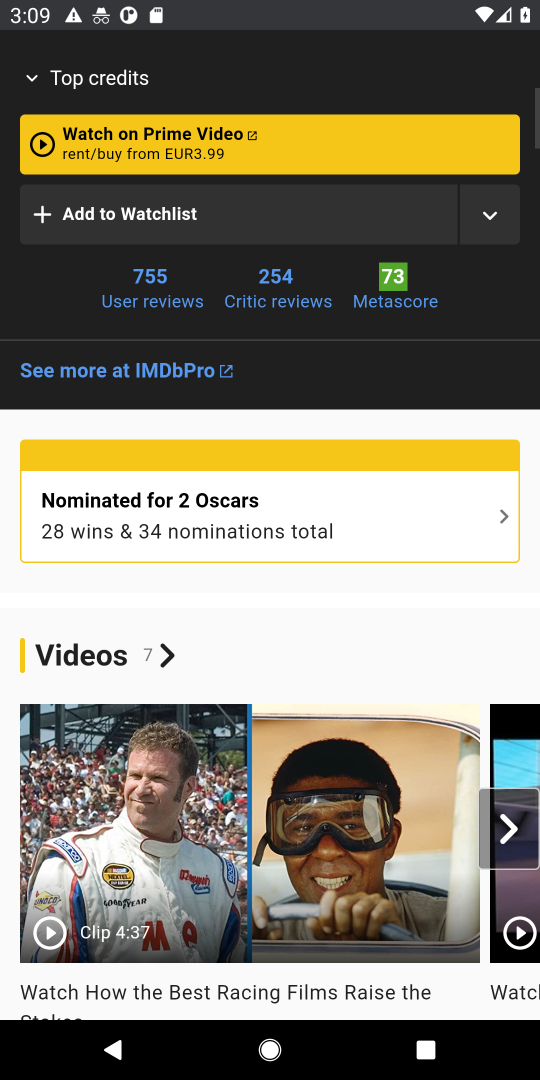
Step 49: drag from (411, 749) to (438, 419)
Your task to perform on an android device: Open a new incognito window in Chrome Image 50: 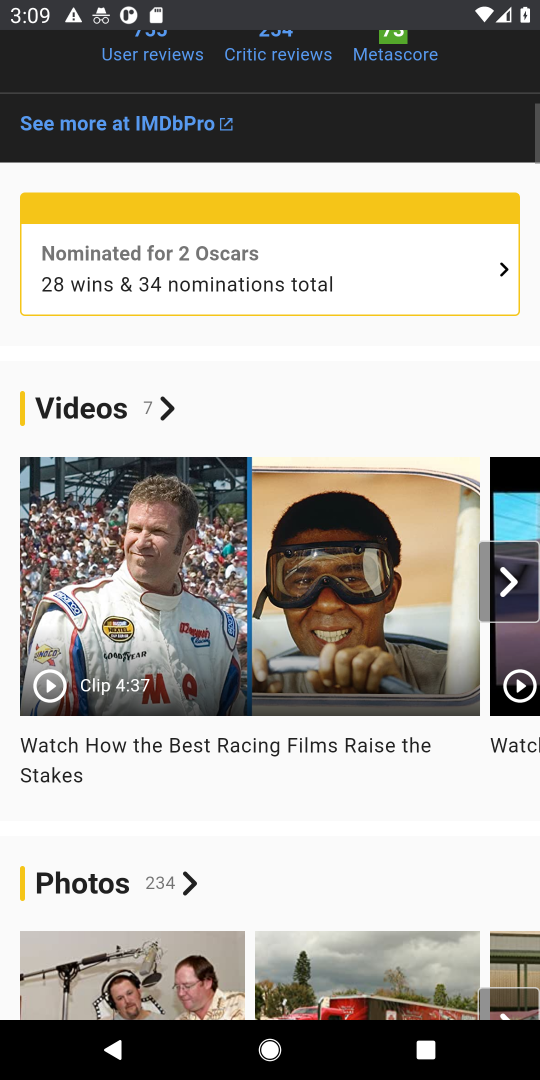
Step 50: drag from (440, 688) to (509, 259)
Your task to perform on an android device: Open a new incognito window in Chrome Image 51: 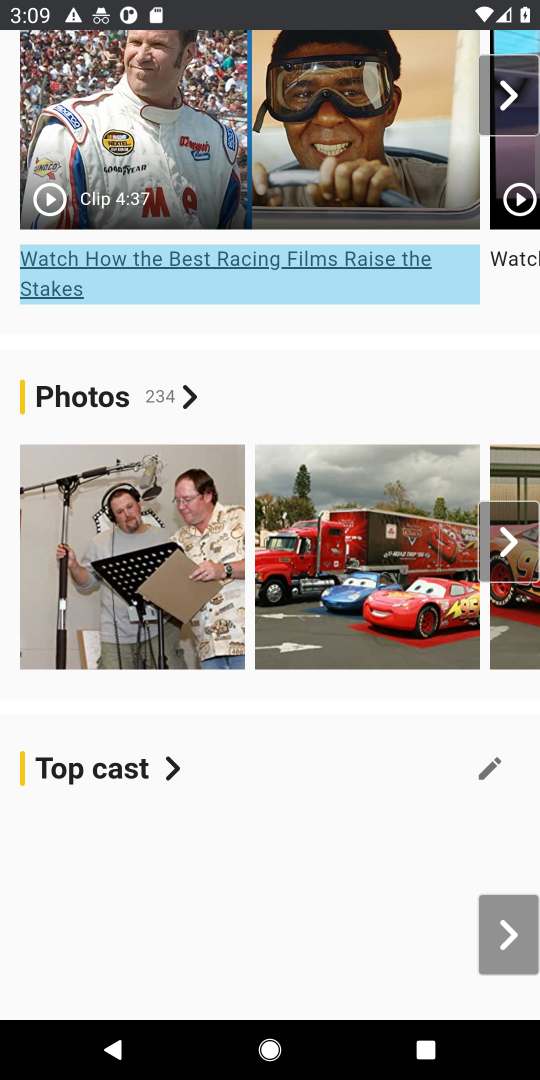
Step 51: drag from (403, 490) to (422, 181)
Your task to perform on an android device: Open a new incognito window in Chrome Image 52: 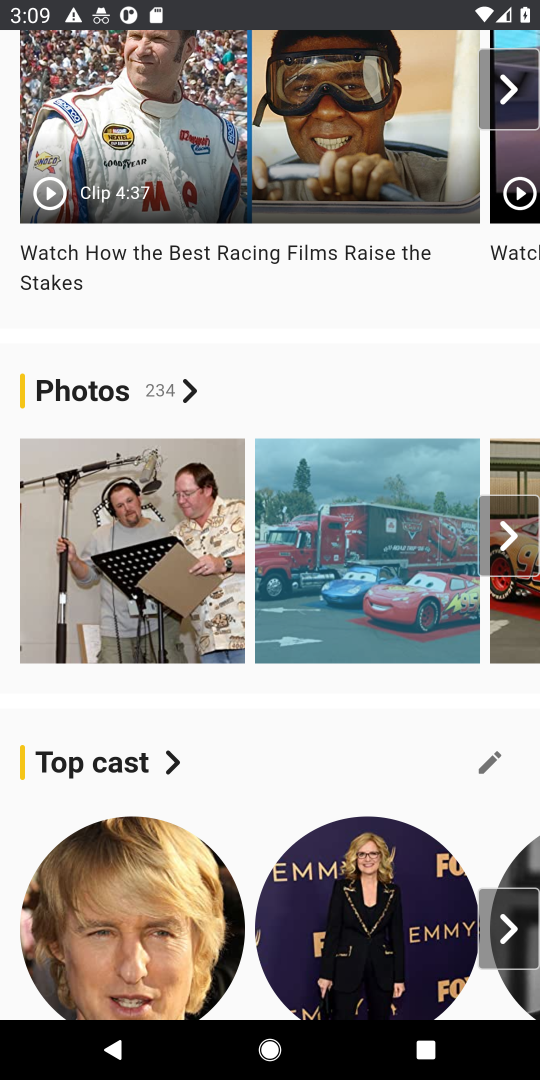
Step 52: drag from (322, 317) to (327, 255)
Your task to perform on an android device: Open a new incognito window in Chrome Image 53: 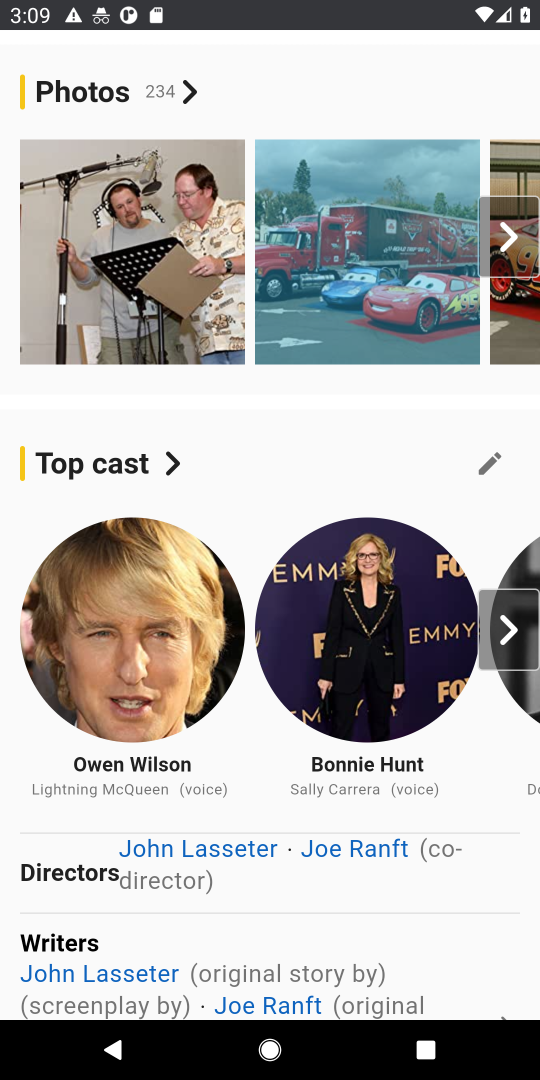
Step 53: drag from (359, 630) to (367, 309)
Your task to perform on an android device: Open a new incognito window in Chrome Image 54: 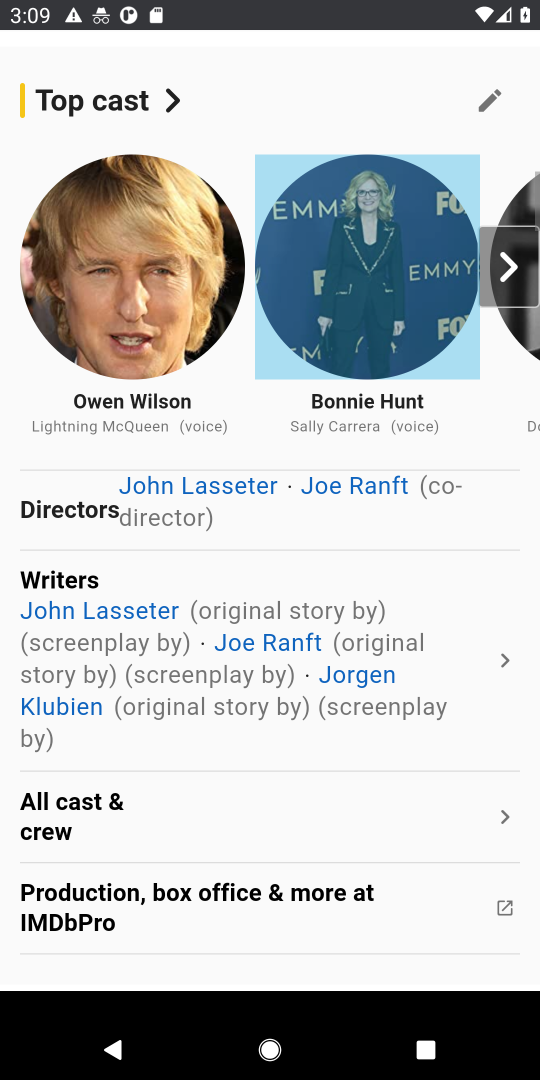
Step 54: click (399, 212)
Your task to perform on an android device: Open a new incognito window in Chrome Image 55: 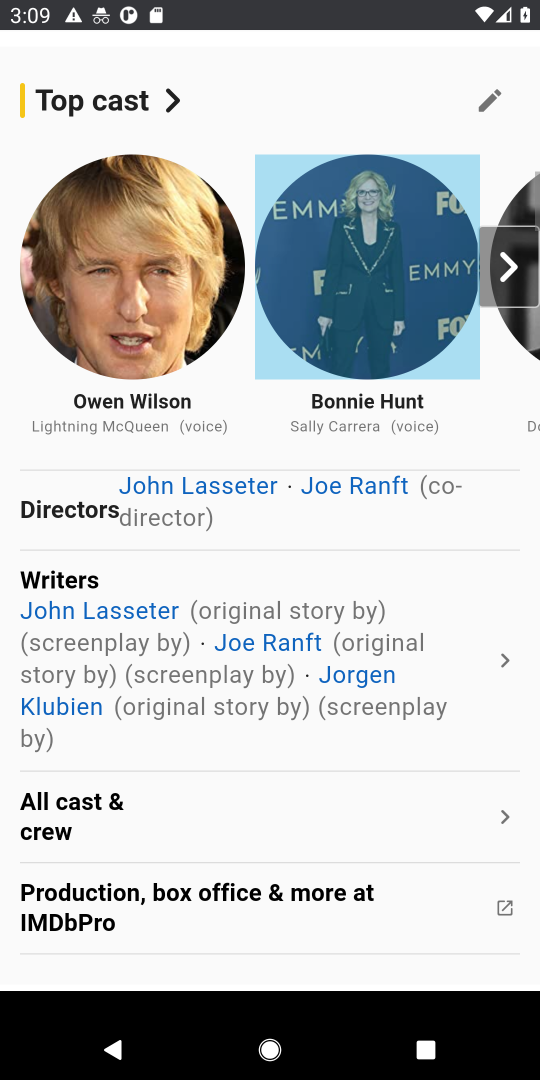
Step 55: drag from (402, 482) to (441, 216)
Your task to perform on an android device: Open a new incognito window in Chrome Image 56: 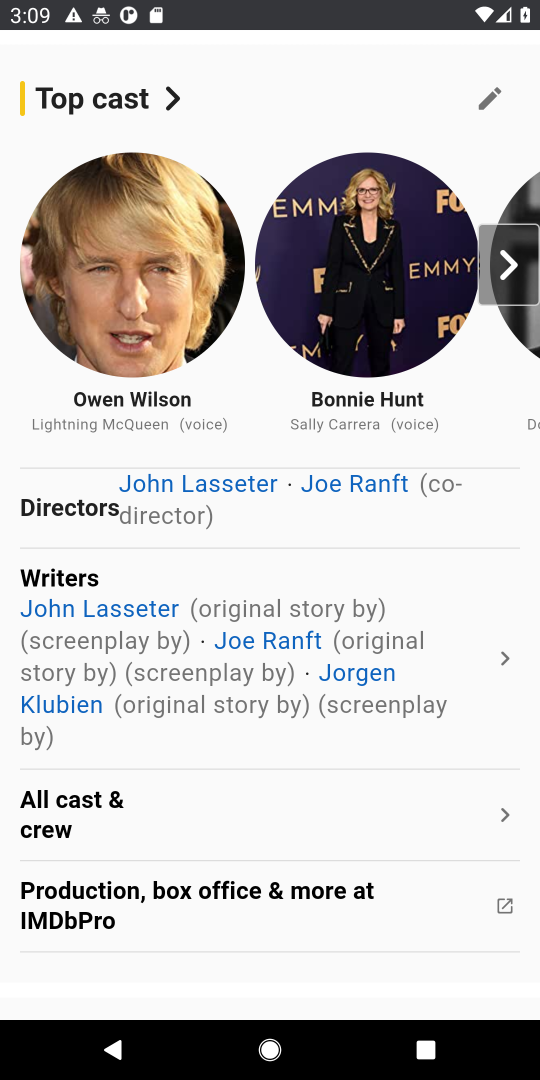
Step 56: drag from (351, 798) to (403, 186)
Your task to perform on an android device: Open a new incognito window in Chrome Image 57: 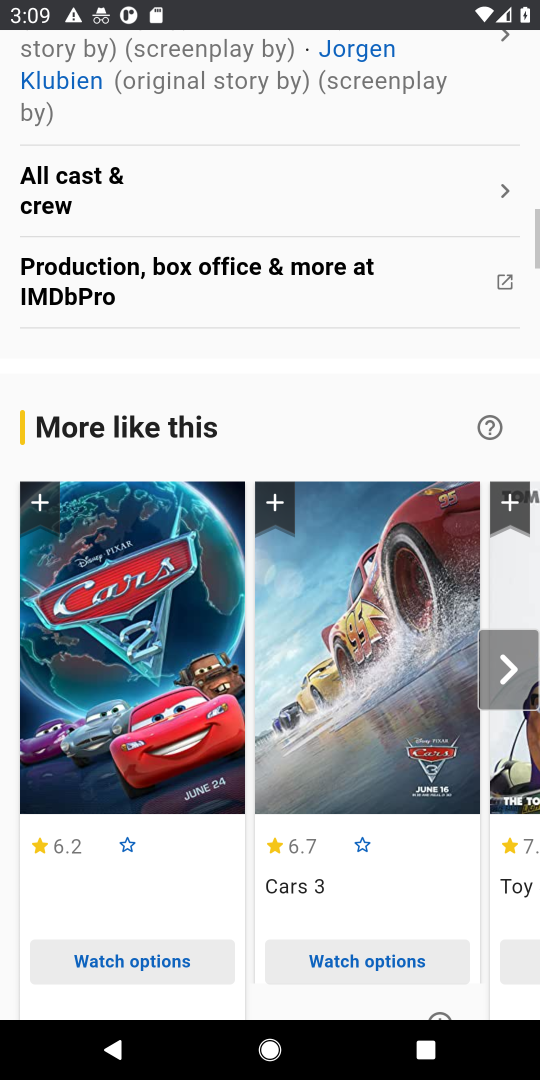
Step 57: drag from (384, 419) to (429, 136)
Your task to perform on an android device: Open a new incognito window in Chrome Image 58: 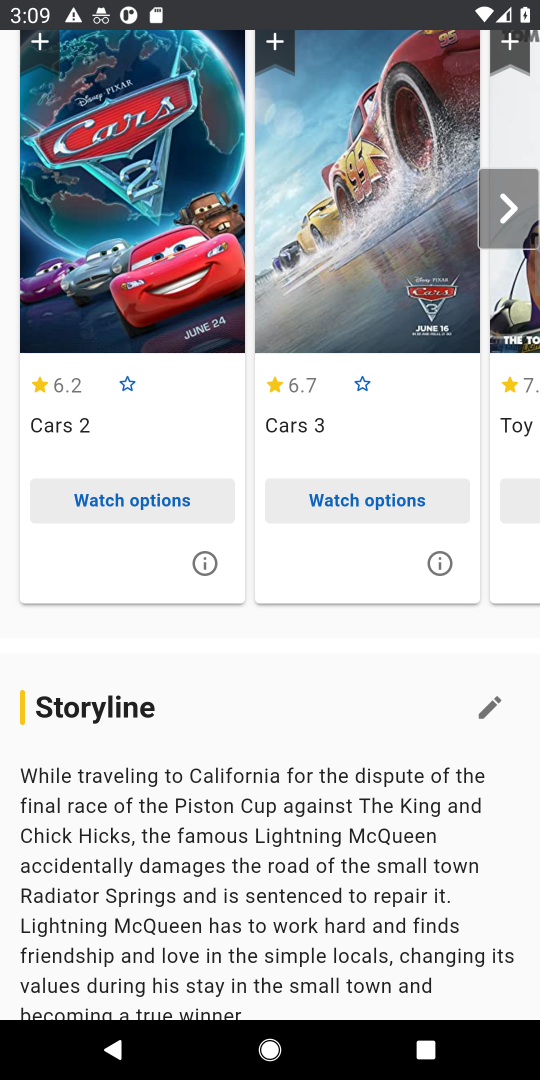
Step 58: drag from (376, 212) to (425, 89)
Your task to perform on an android device: Open a new incognito window in Chrome Image 59: 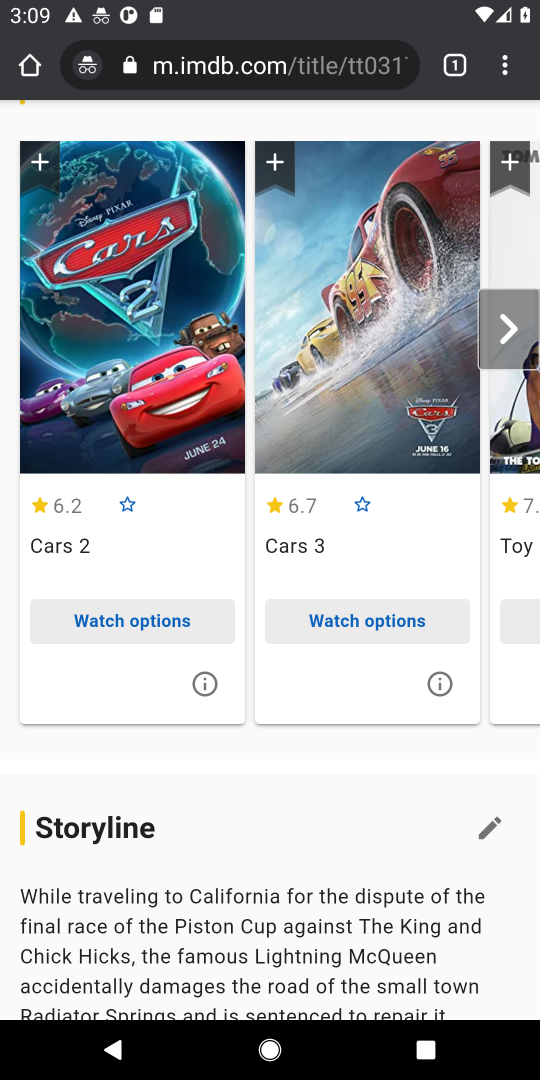
Step 59: drag from (430, 670) to (500, 256)
Your task to perform on an android device: Open a new incognito window in Chrome Image 60: 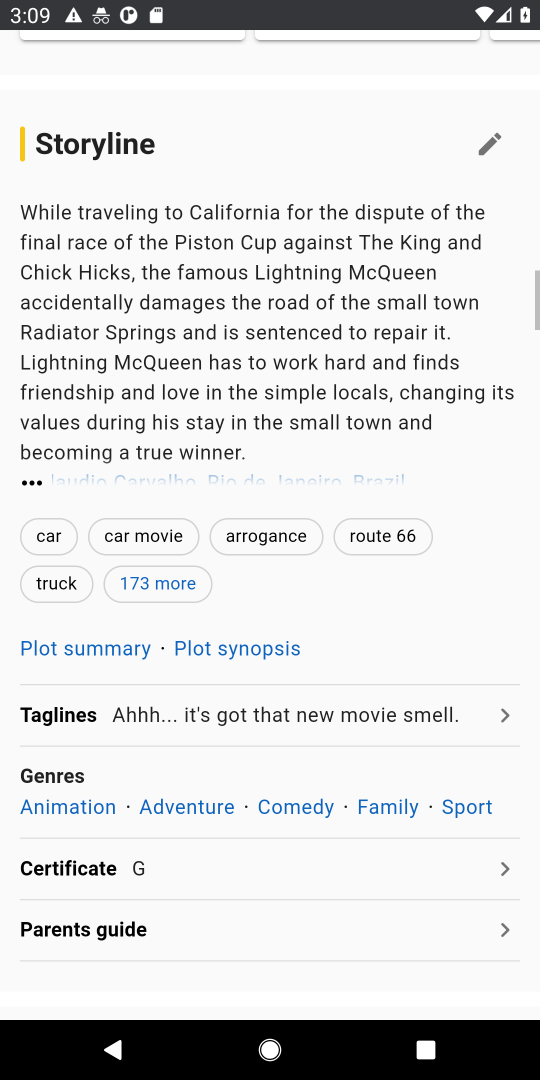
Step 60: drag from (477, 418) to (494, 243)
Your task to perform on an android device: Open a new incognito window in Chrome Image 61: 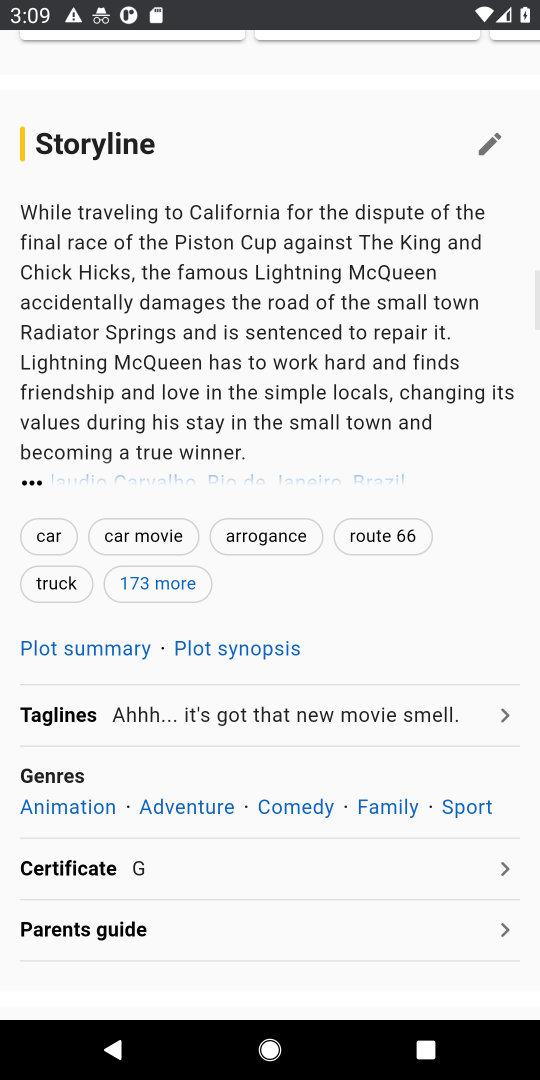
Step 61: drag from (452, 538) to (466, 204)
Your task to perform on an android device: Open a new incognito window in Chrome Image 62: 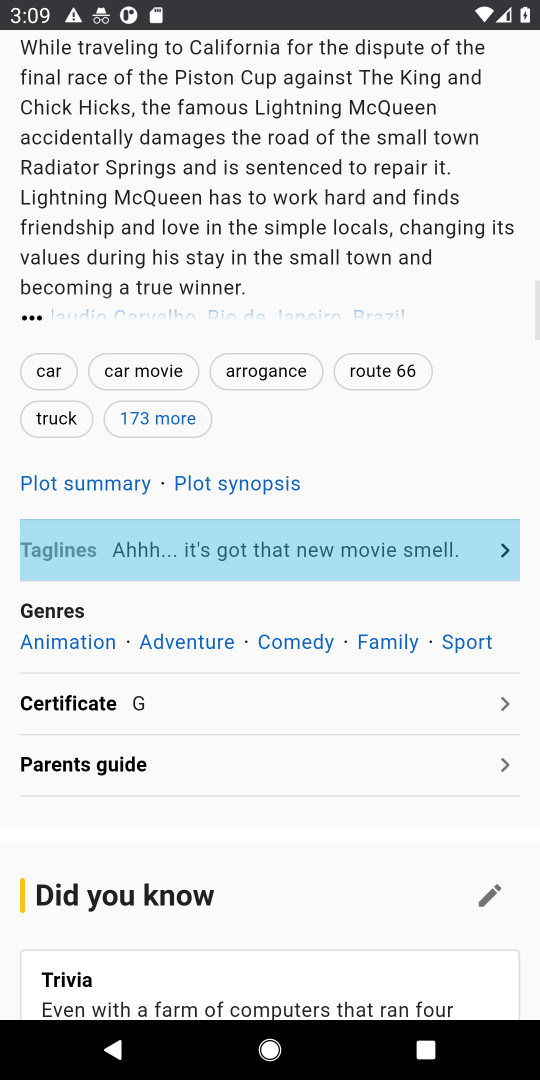
Step 62: drag from (460, 380) to (411, 281)
Your task to perform on an android device: Open a new incognito window in Chrome Image 63: 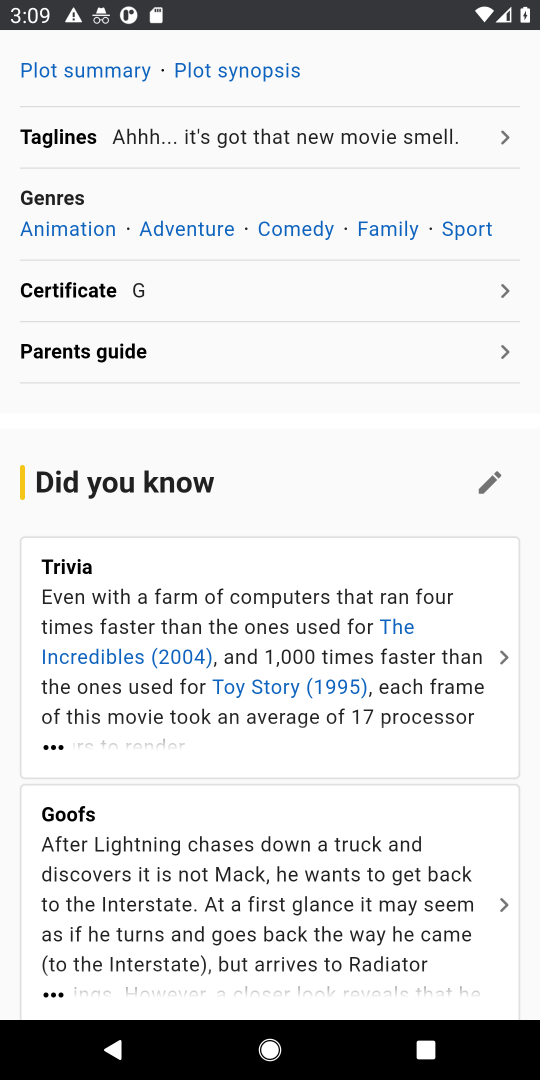
Step 63: drag from (357, 669) to (379, 257)
Your task to perform on an android device: Open a new incognito window in Chrome Image 64: 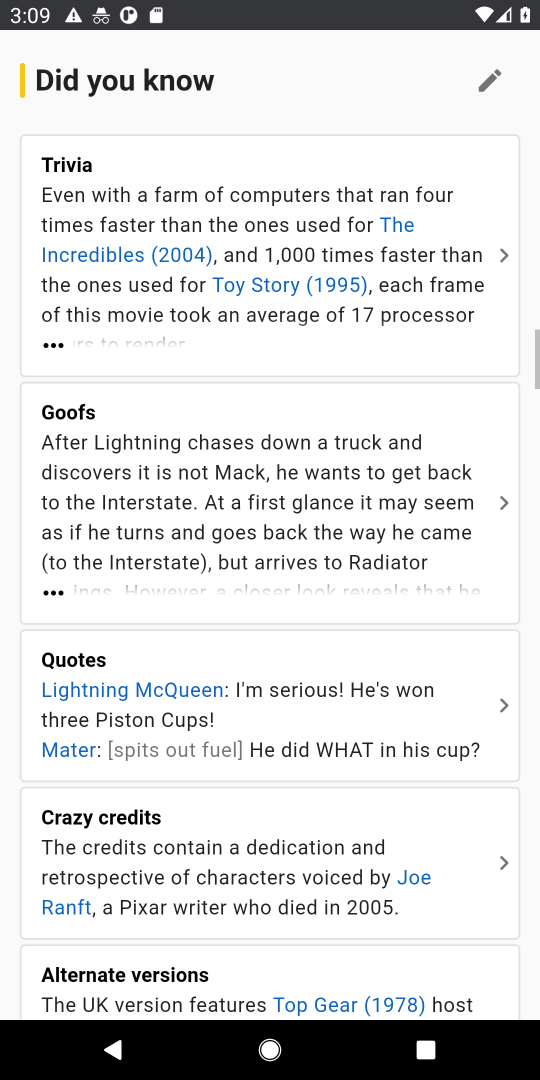
Step 64: drag from (391, 780) to (417, 195)
Your task to perform on an android device: Open a new incognito window in Chrome Image 65: 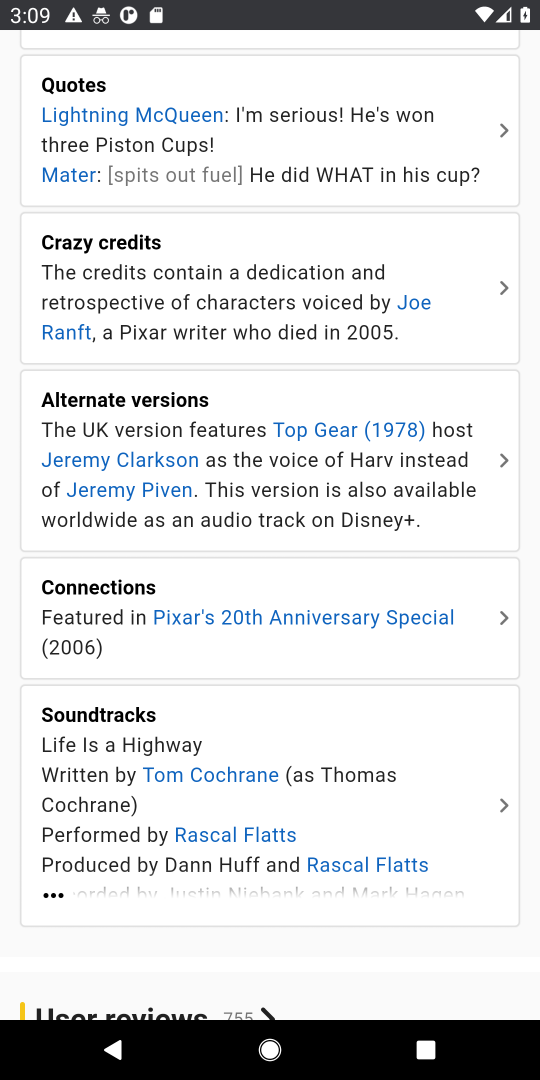
Step 65: press back button
Your task to perform on an android device: Open a new incognito window in Chrome Image 66: 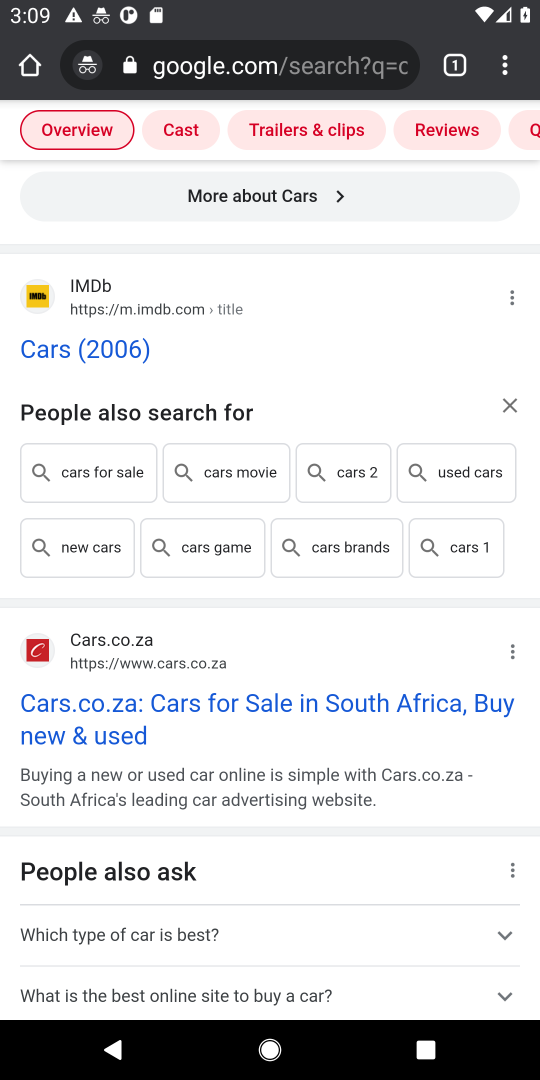
Step 66: click (227, 714)
Your task to perform on an android device: Open a new incognito window in Chrome Image 67: 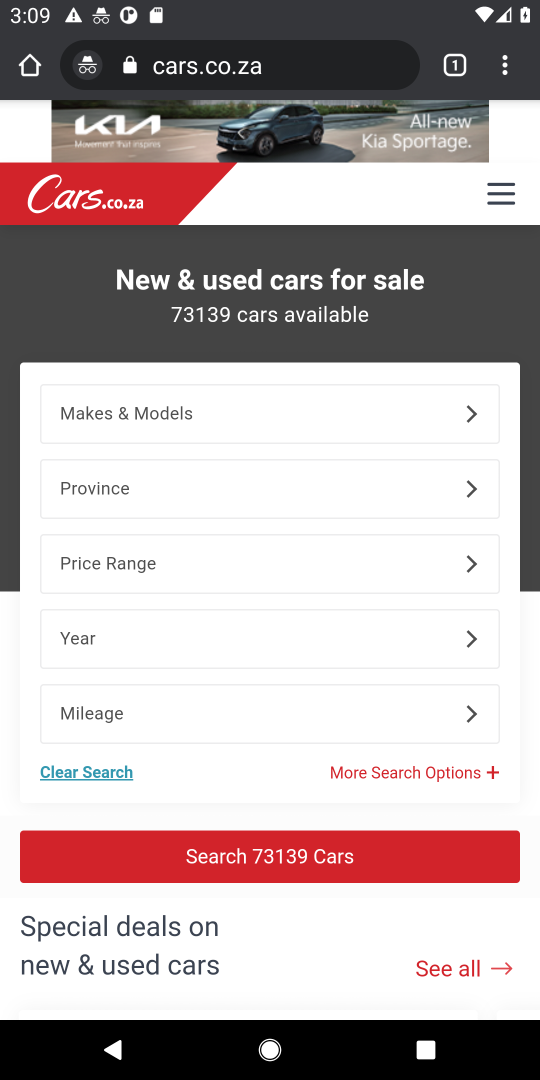
Step 67: drag from (285, 940) to (409, 218)
Your task to perform on an android device: Open a new incognito window in Chrome Image 68: 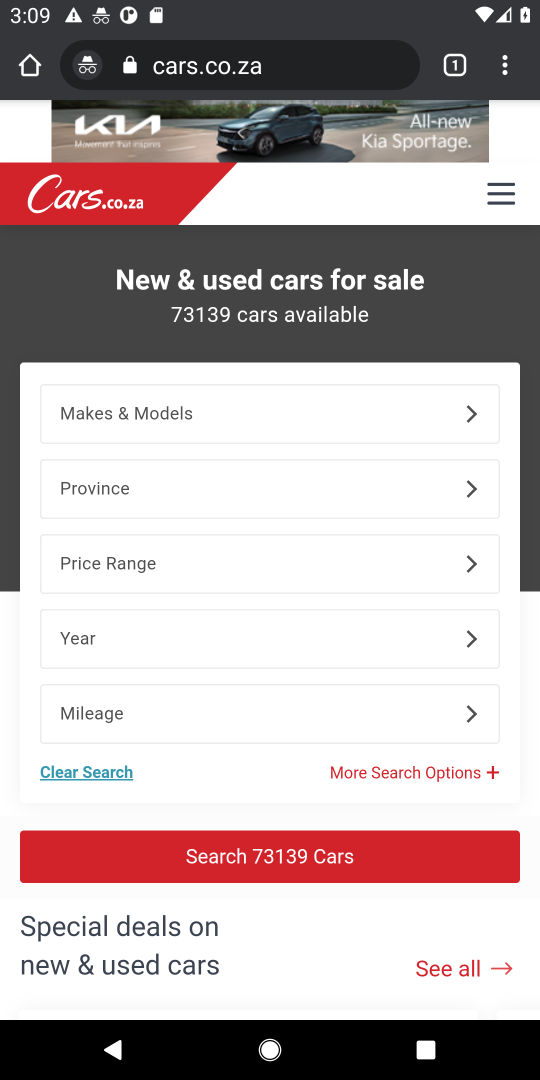
Step 68: drag from (375, 951) to (390, 291)
Your task to perform on an android device: Open a new incognito window in Chrome Image 69: 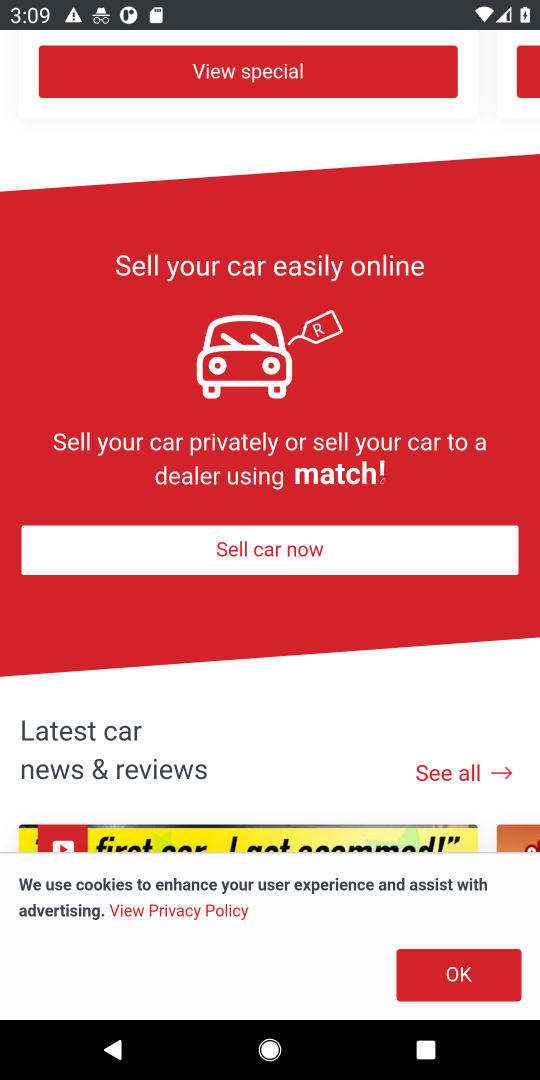
Step 69: drag from (346, 557) to (349, 751)
Your task to perform on an android device: Open a new incognito window in Chrome Image 70: 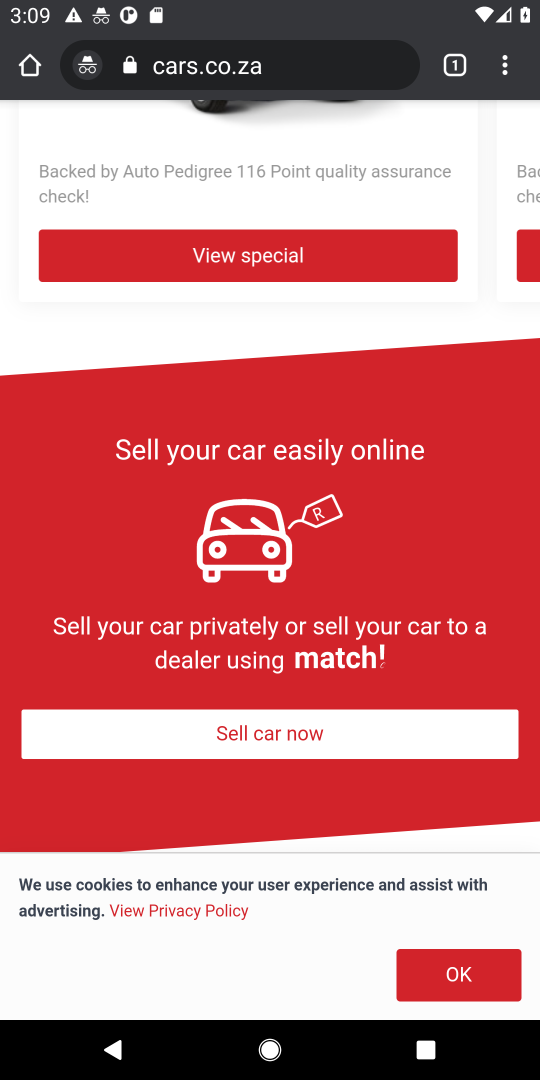
Step 70: drag from (361, 521) to (386, 900)
Your task to perform on an android device: Open a new incognito window in Chrome Image 71: 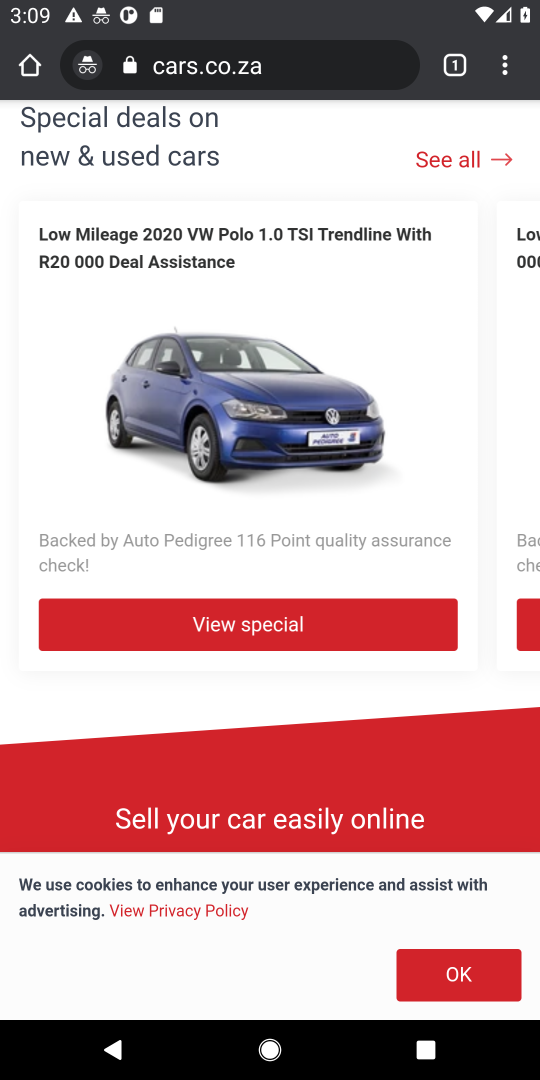
Step 71: drag from (462, 479) to (103, 492)
Your task to perform on an android device: Open a new incognito window in Chrome Image 72: 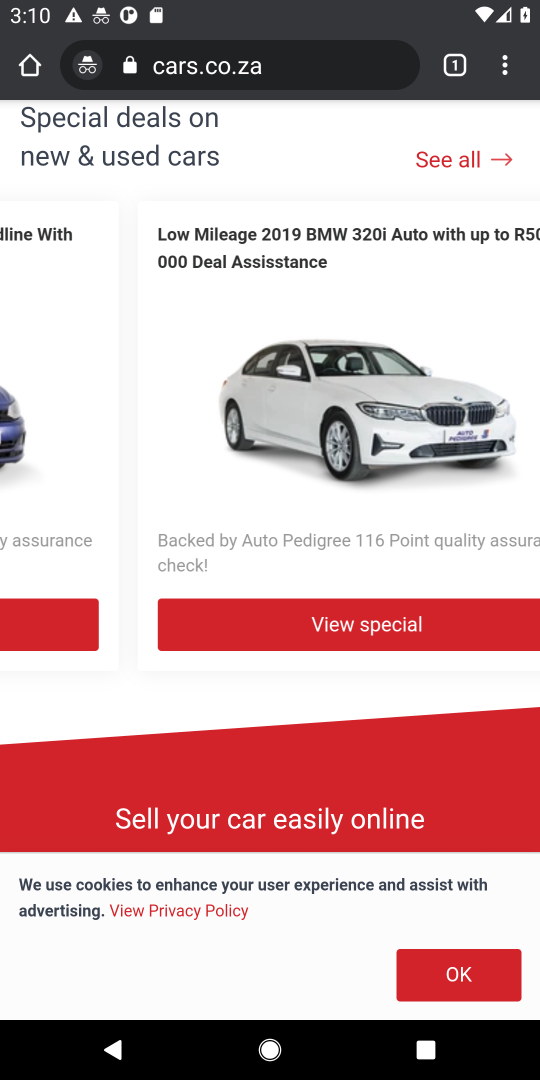
Step 72: drag from (365, 481) to (82, 501)
Your task to perform on an android device: Open a new incognito window in Chrome Image 73: 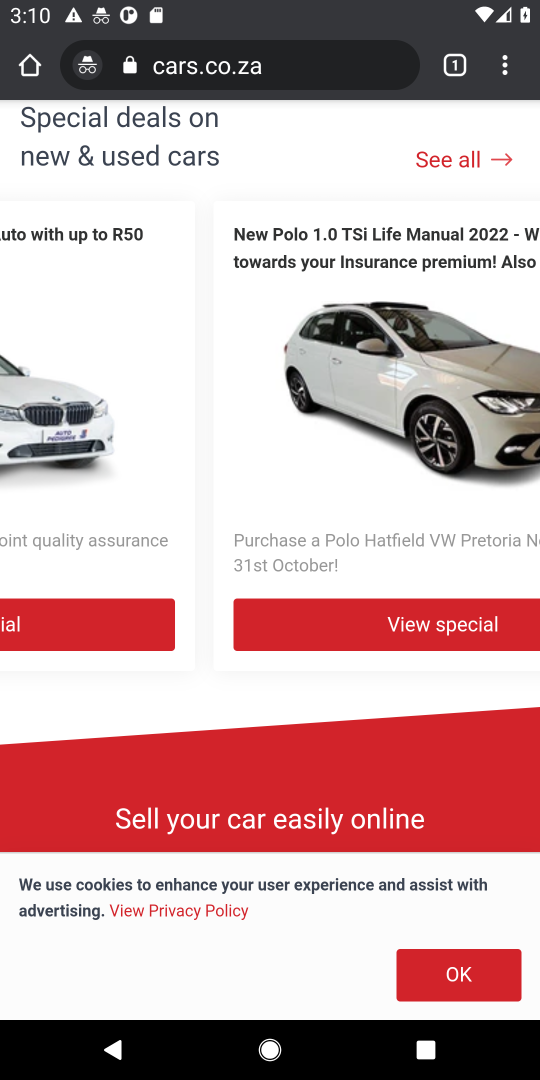
Step 73: drag from (525, 479) to (0, 470)
Your task to perform on an android device: Open a new incognito window in Chrome Image 74: 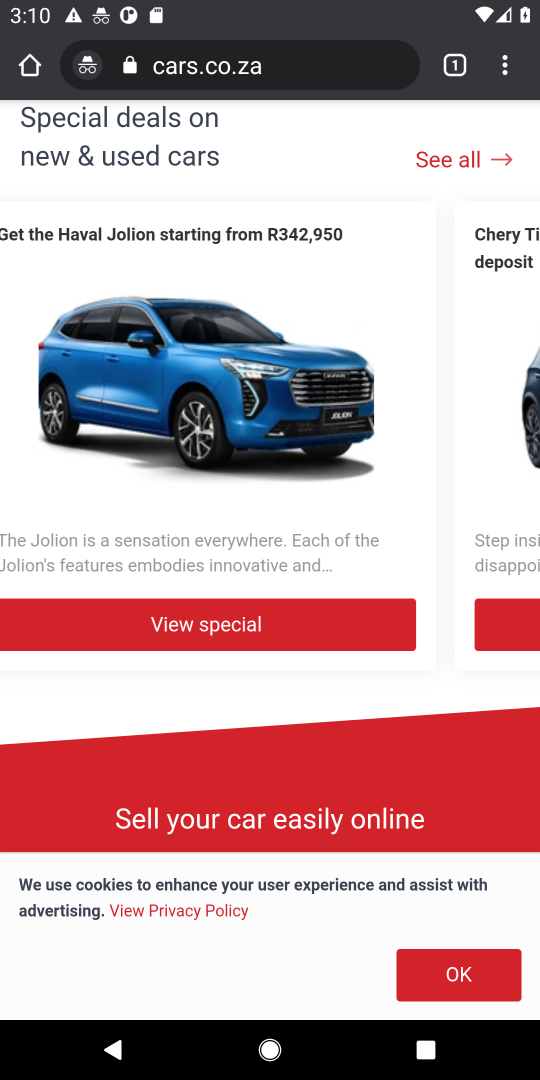
Step 74: drag from (463, 472) to (10, 492)
Your task to perform on an android device: Open a new incognito window in Chrome Image 75: 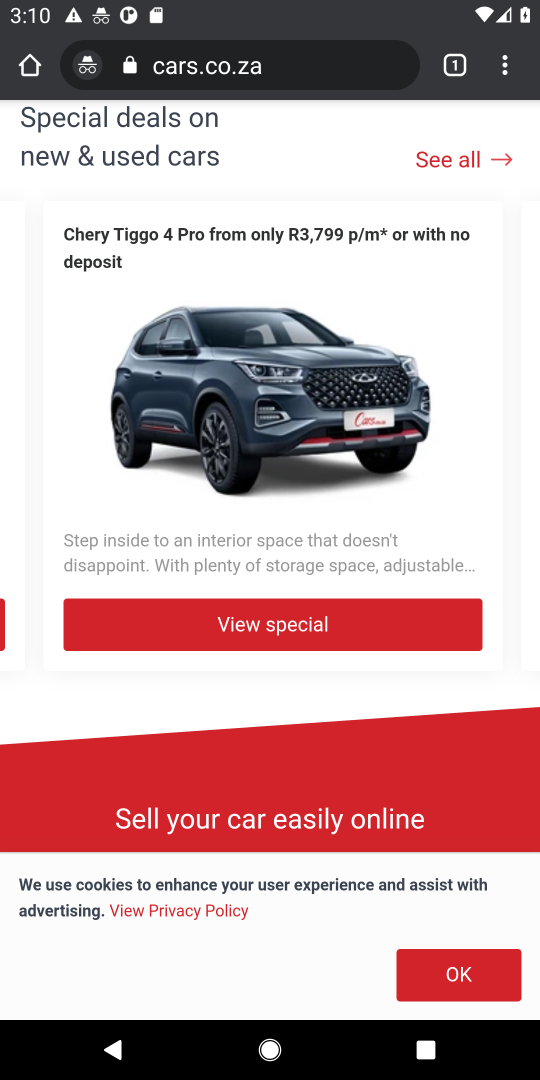
Step 75: drag from (491, 462) to (0, 504)
Your task to perform on an android device: Open a new incognito window in Chrome Image 76: 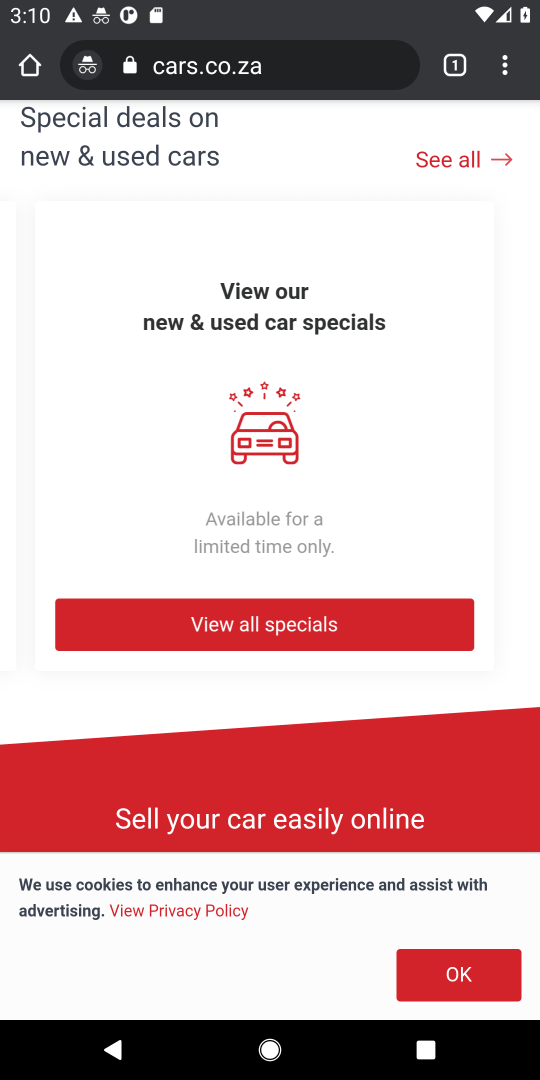
Step 76: drag from (226, 464) to (532, 428)
Your task to perform on an android device: Open a new incognito window in Chrome Image 77: 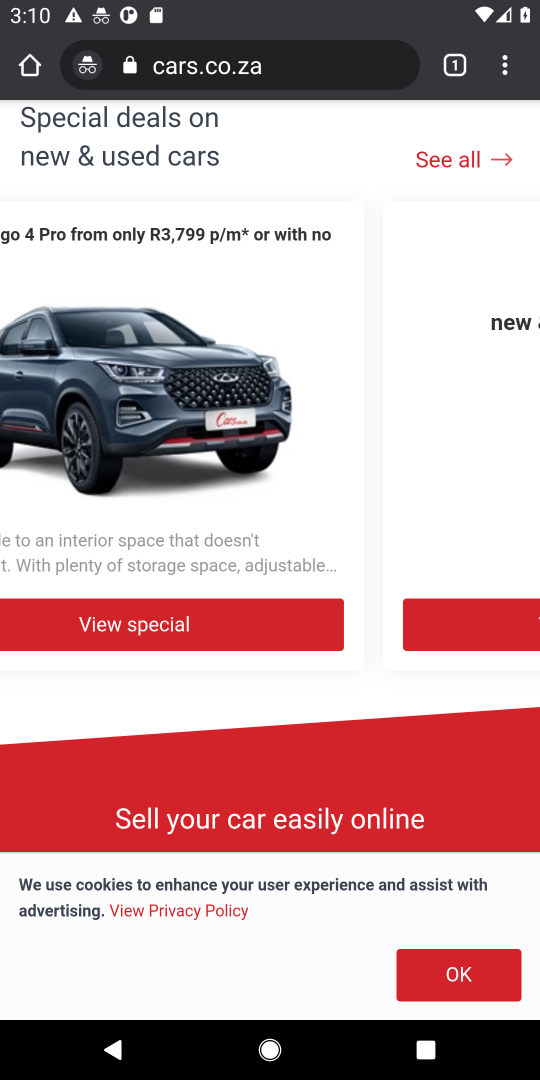
Step 77: drag from (139, 421) to (535, 425)
Your task to perform on an android device: Open a new incognito window in Chrome Image 78: 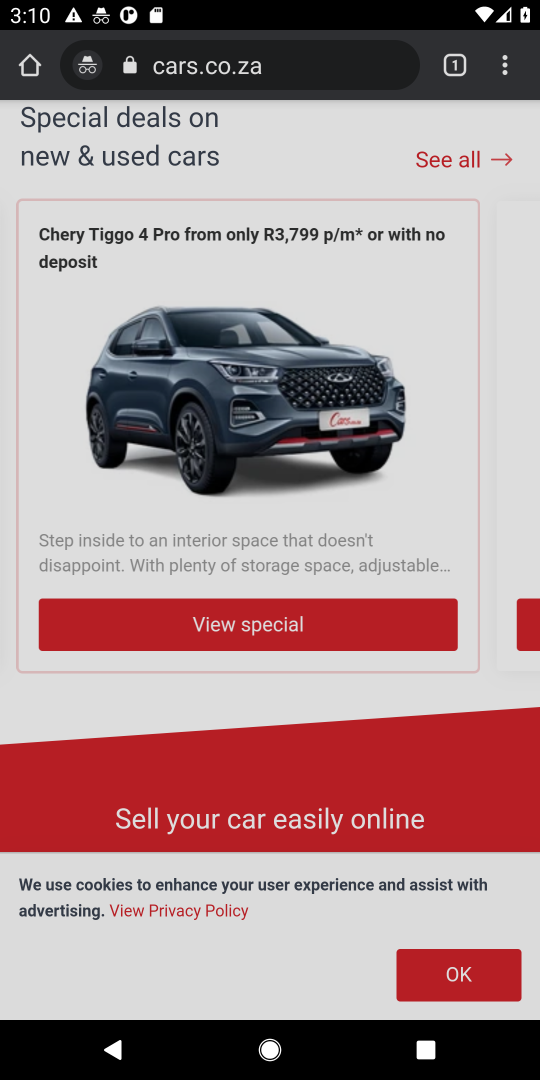
Step 78: drag from (72, 425) to (516, 460)
Your task to perform on an android device: Open a new incognito window in Chrome Image 79: 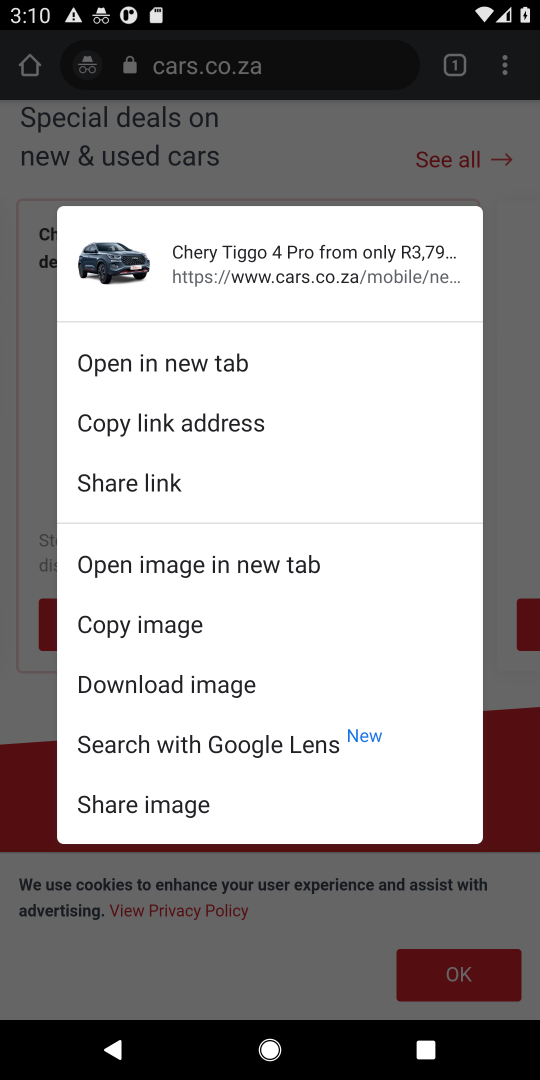
Step 79: click (323, 148)
Your task to perform on an android device: Open a new incognito window in Chrome Image 80: 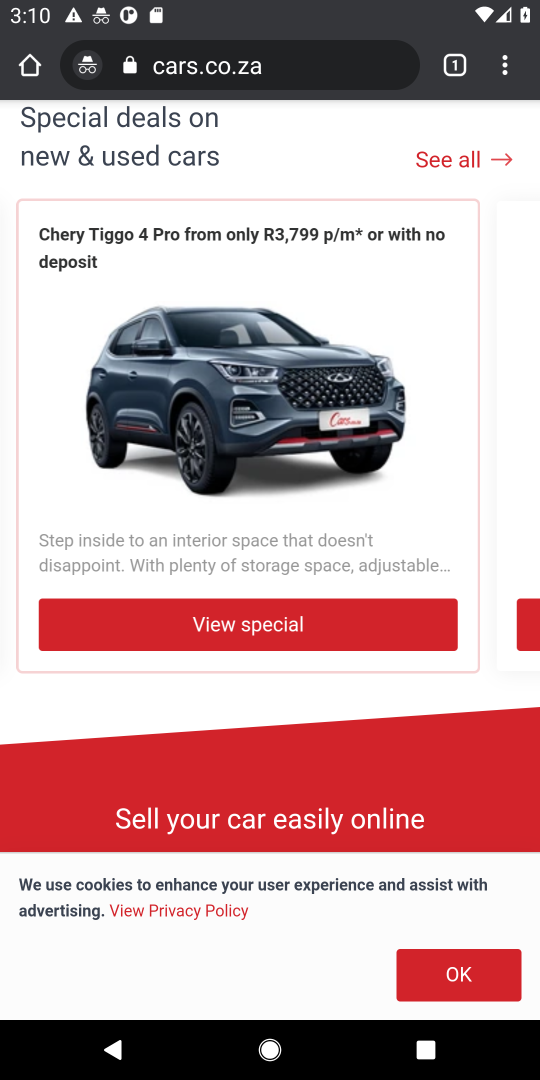
Step 80: drag from (56, 422) to (517, 441)
Your task to perform on an android device: Open a new incognito window in Chrome Image 81: 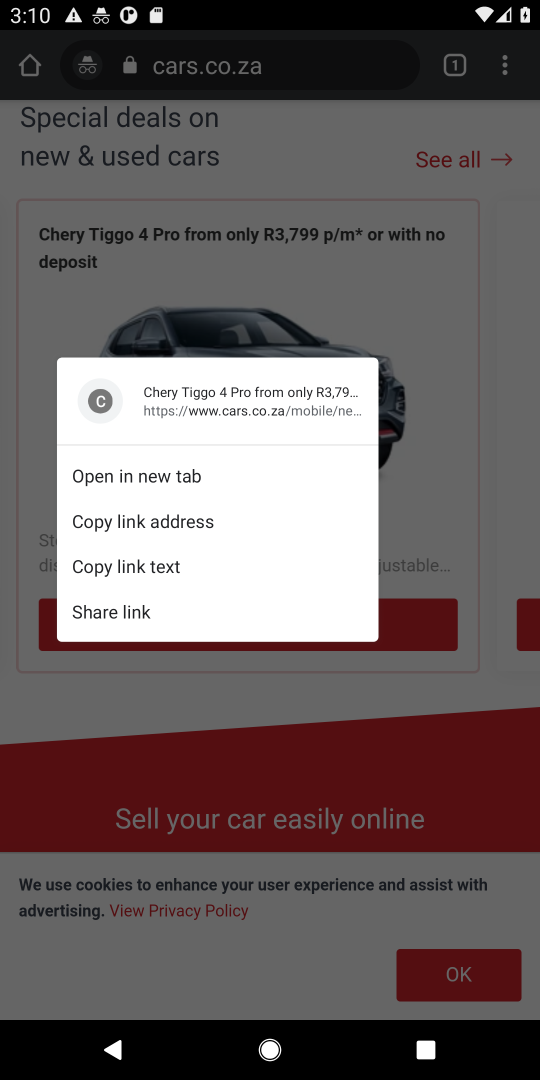
Step 81: drag from (202, 430) to (537, 443)
Your task to perform on an android device: Open a new incognito window in Chrome Image 82: 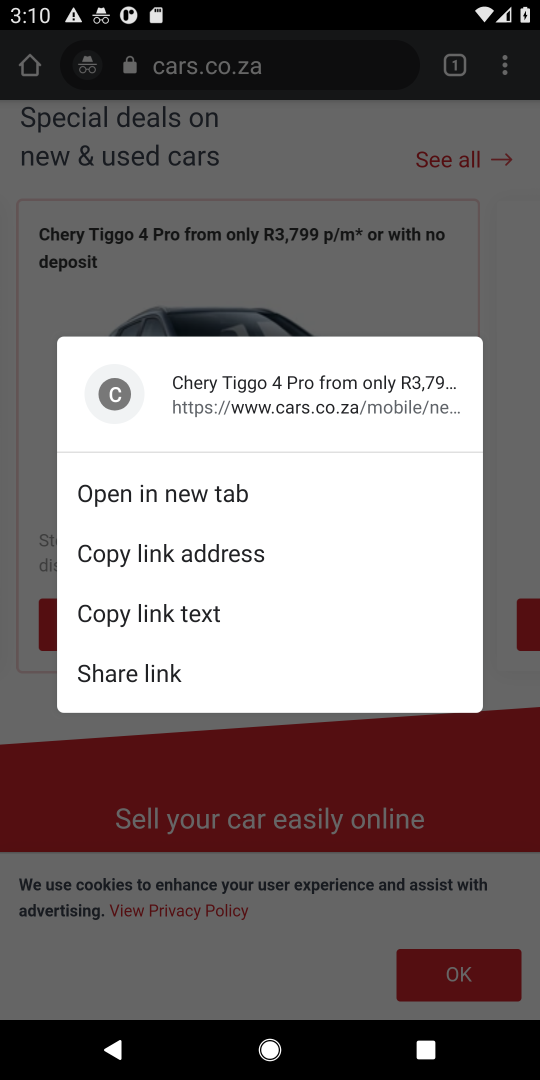
Step 82: click (380, 201)
Your task to perform on an android device: Open a new incognito window in Chrome Image 83: 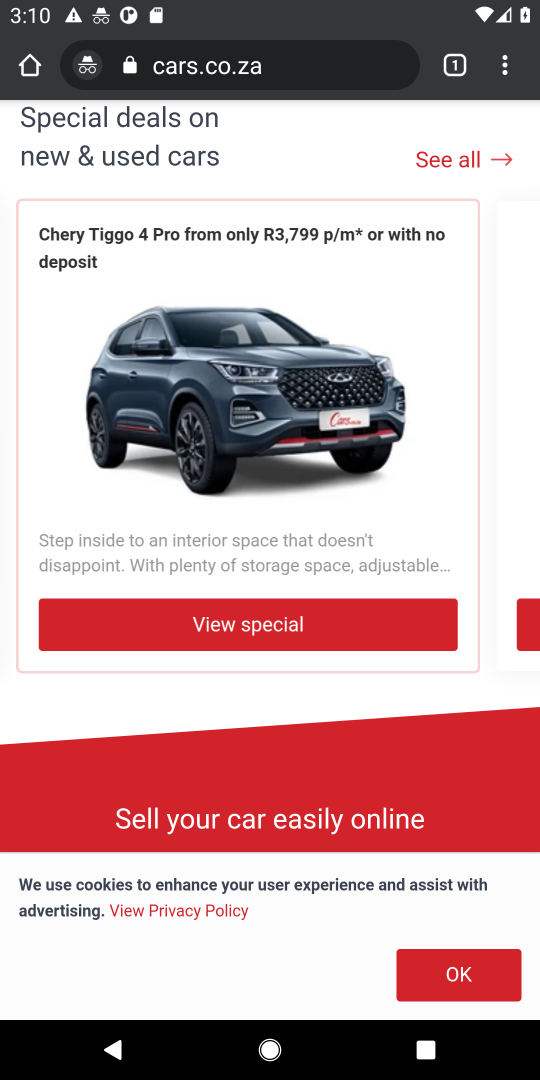
Step 83: drag from (95, 402) to (509, 424)
Your task to perform on an android device: Open a new incognito window in Chrome Image 84: 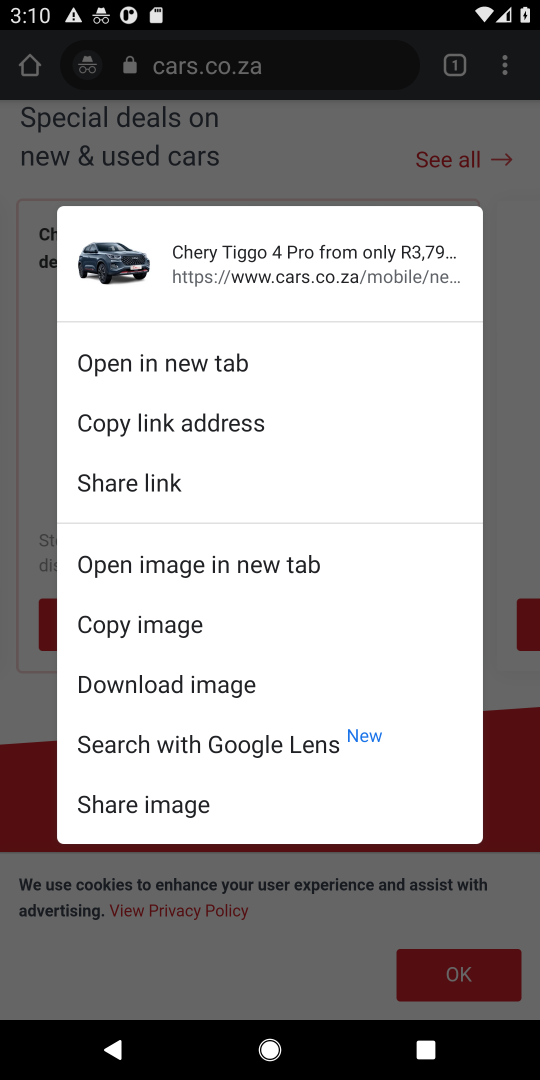
Step 84: click (375, 140)
Your task to perform on an android device: Open a new incognito window in Chrome Image 85: 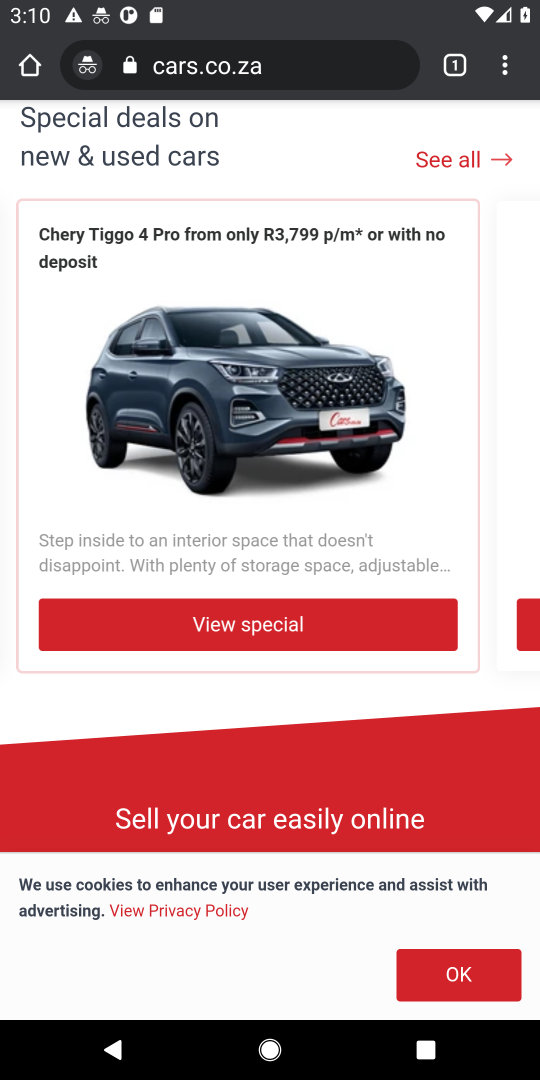
Step 85: drag from (376, 466) to (161, 468)
Your task to perform on an android device: Open a new incognito window in Chrome Image 86: 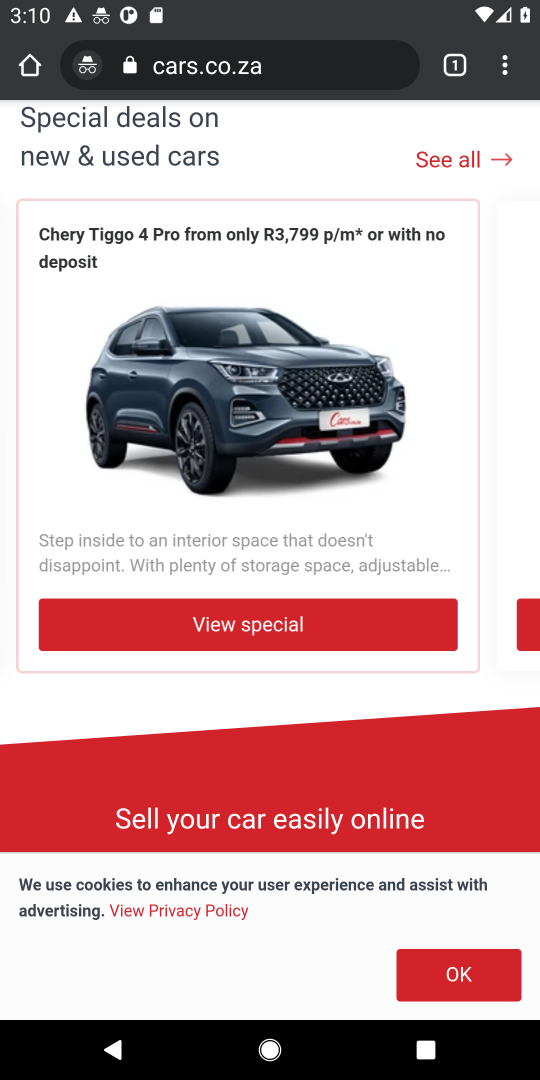
Step 86: press back button
Your task to perform on an android device: Open a new incognito window in Chrome Image 87: 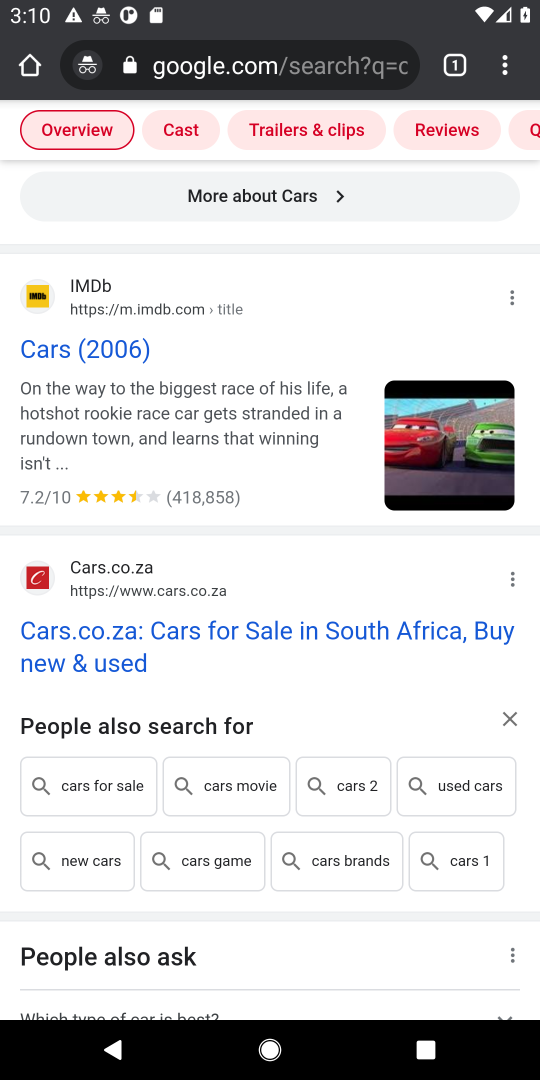
Step 87: click (405, 646)
Your task to perform on an android device: Open a new incognito window in Chrome Image 88: 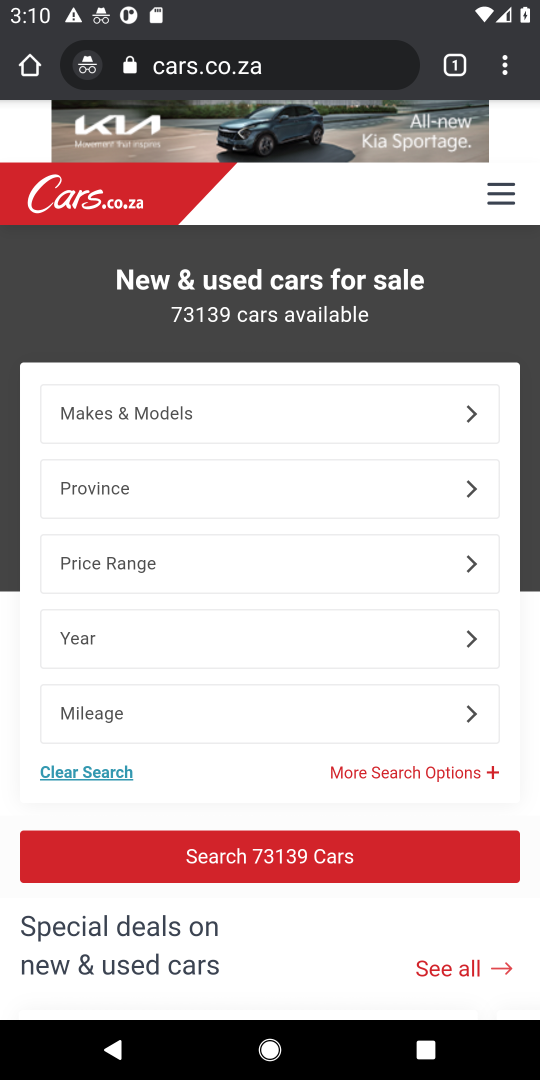
Step 88: drag from (407, 700) to (400, 281)
Your task to perform on an android device: Open a new incognito window in Chrome Image 89: 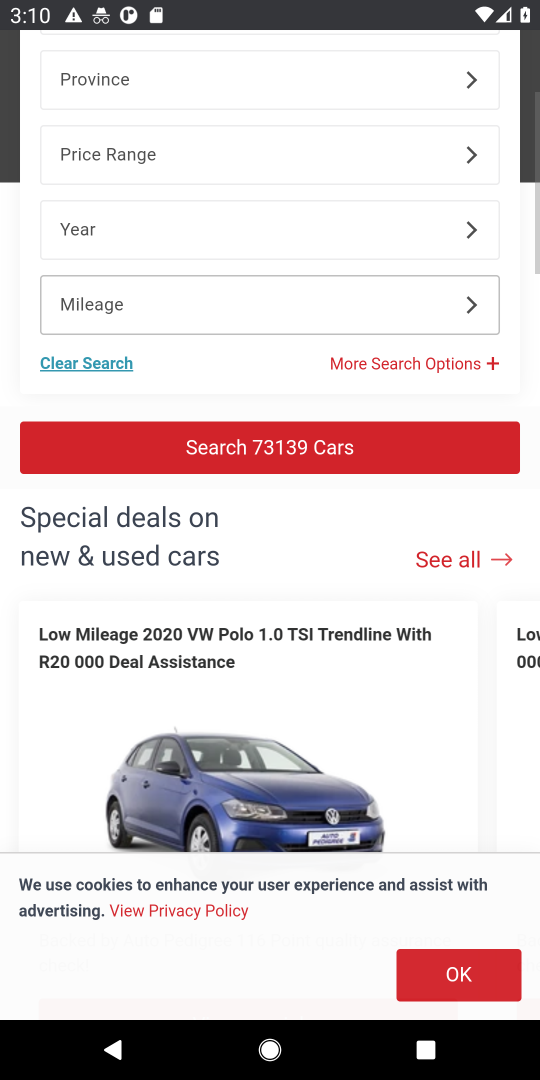
Step 89: drag from (375, 682) to (434, 353)
Your task to perform on an android device: Open a new incognito window in Chrome Image 90: 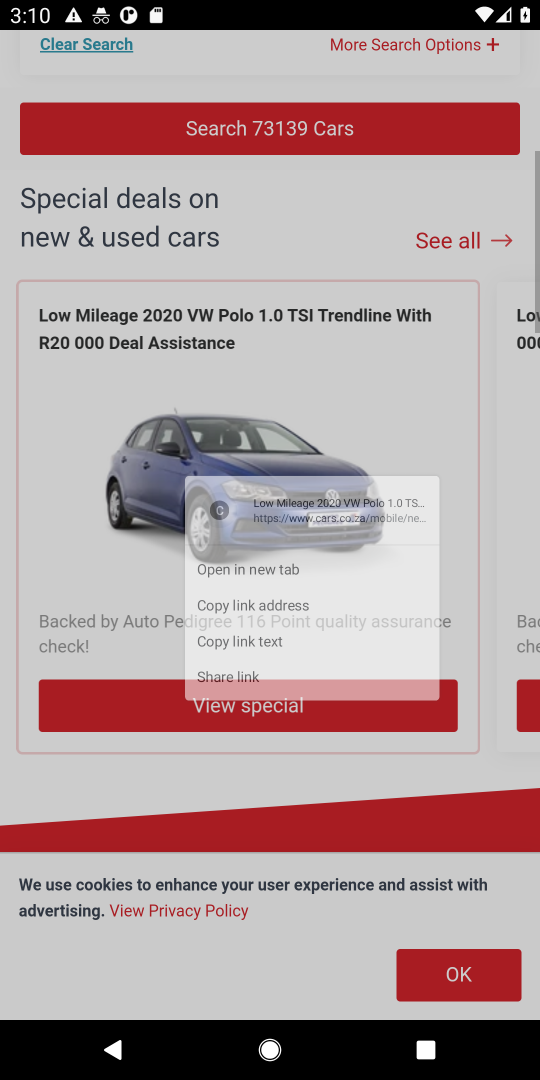
Step 90: drag from (460, 753) to (413, 462)
Your task to perform on an android device: Open a new incognito window in Chrome Image 91: 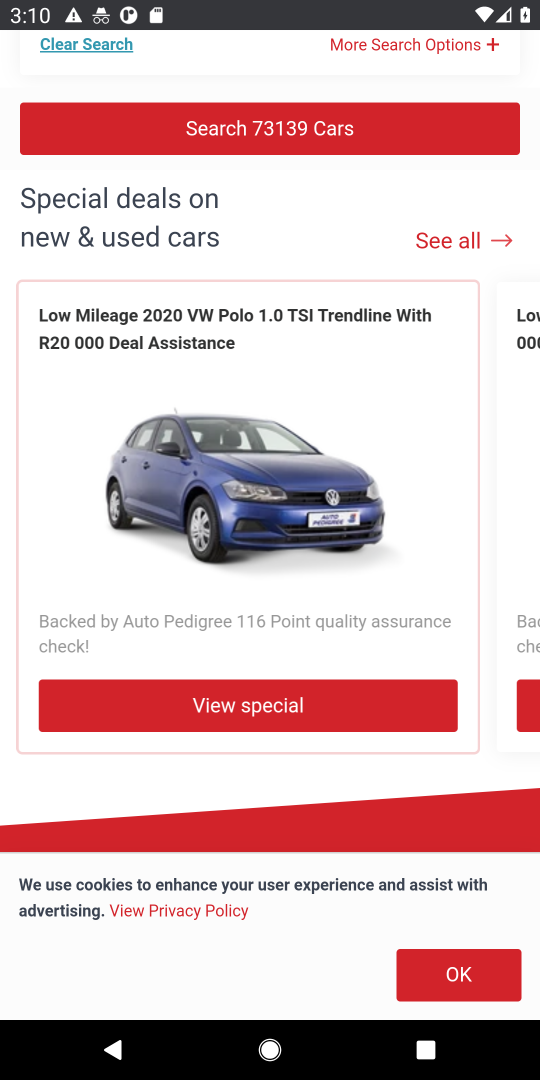
Step 91: drag from (372, 858) to (380, 454)
Your task to perform on an android device: Open a new incognito window in Chrome Image 92: 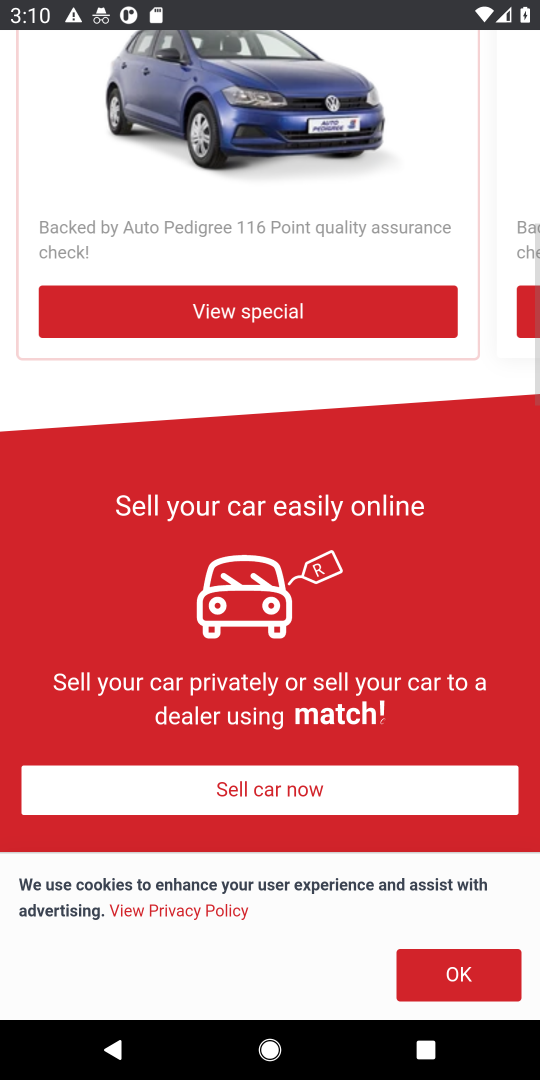
Step 92: drag from (291, 711) to (388, 250)
Your task to perform on an android device: Open a new incognito window in Chrome Image 93: 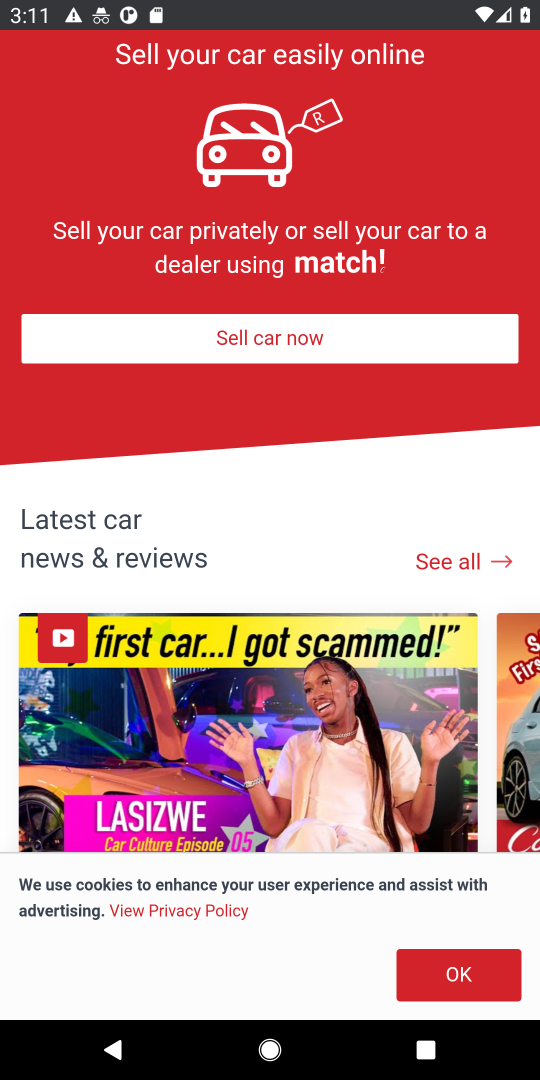
Step 93: drag from (403, 615) to (463, 363)
Your task to perform on an android device: Open a new incognito window in Chrome Image 94: 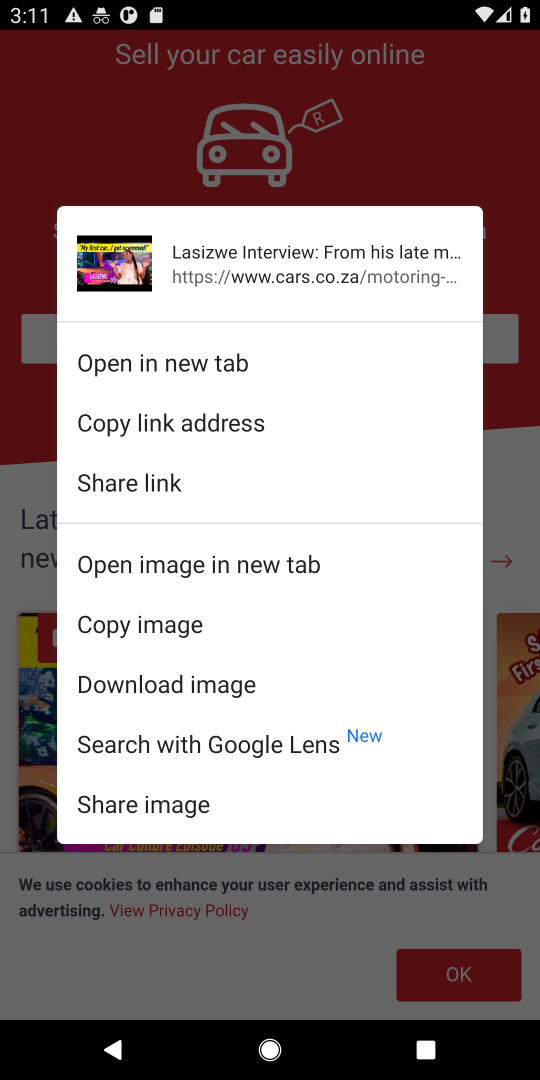
Step 94: drag from (437, 570) to (456, 301)
Your task to perform on an android device: Open a new incognito window in Chrome Image 95: 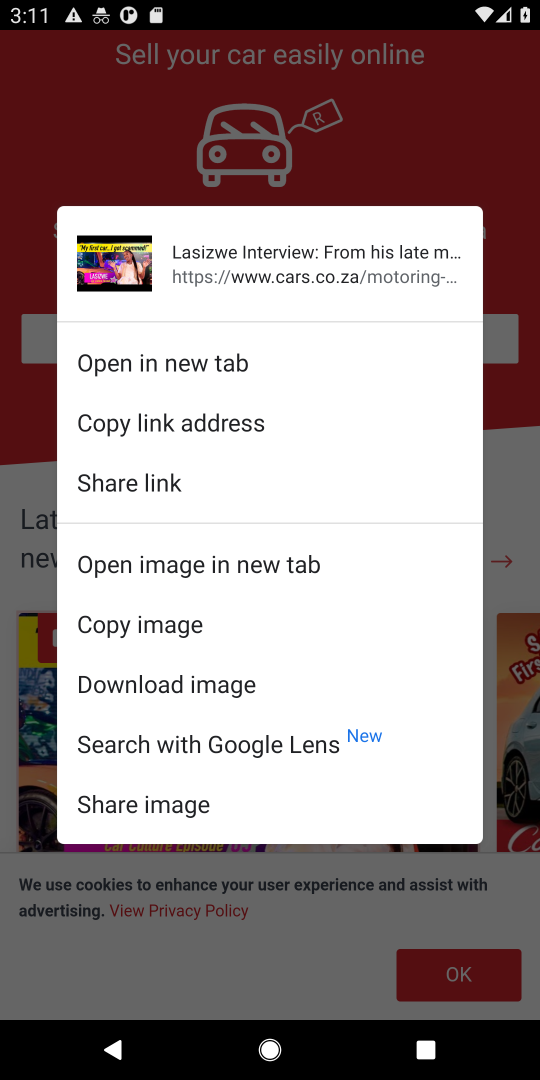
Step 95: drag from (417, 736) to (431, 443)
Your task to perform on an android device: Open a new incognito window in Chrome Image 96: 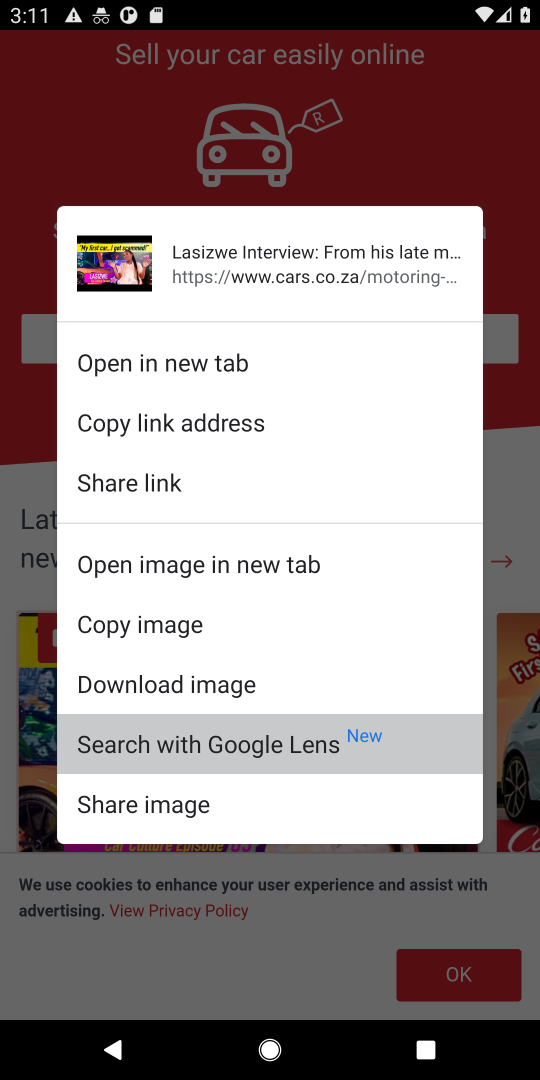
Step 96: click (467, 150)
Your task to perform on an android device: Open a new incognito window in Chrome Image 97: 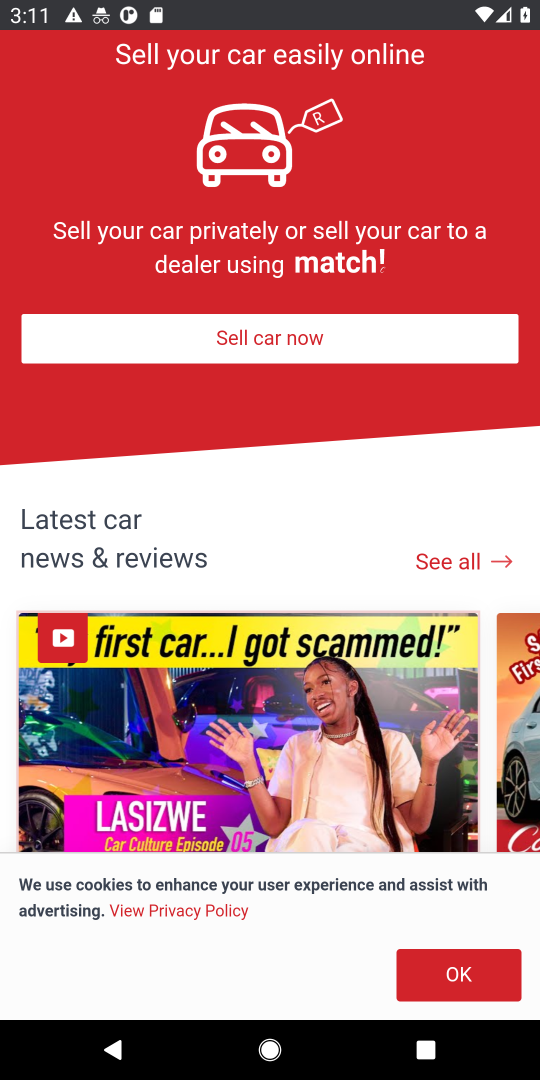
Step 97: drag from (425, 485) to (424, 253)
Your task to perform on an android device: Open a new incognito window in Chrome Image 98: 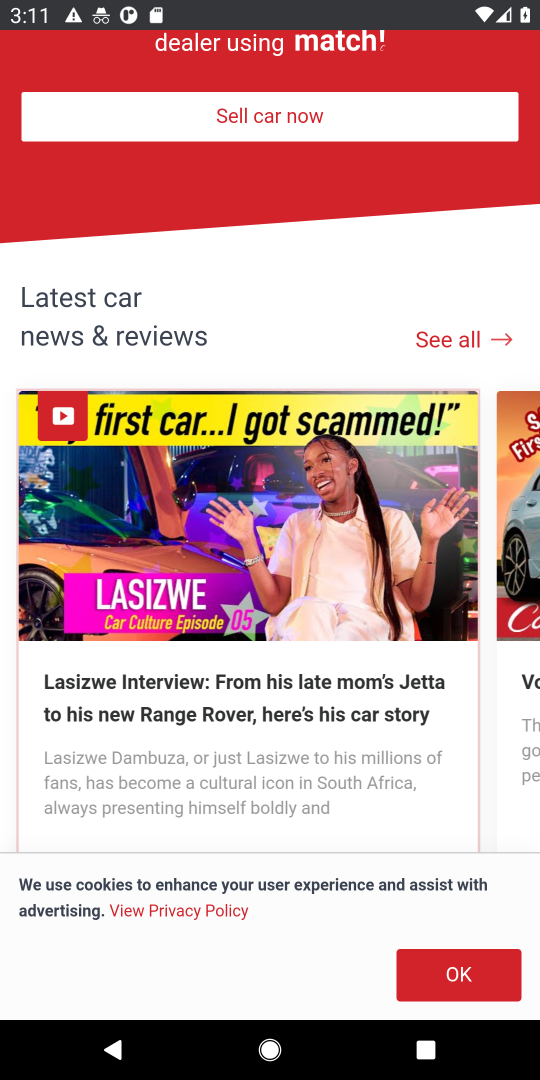
Step 98: drag from (399, 504) to (444, 220)
Your task to perform on an android device: Open a new incognito window in Chrome Image 99: 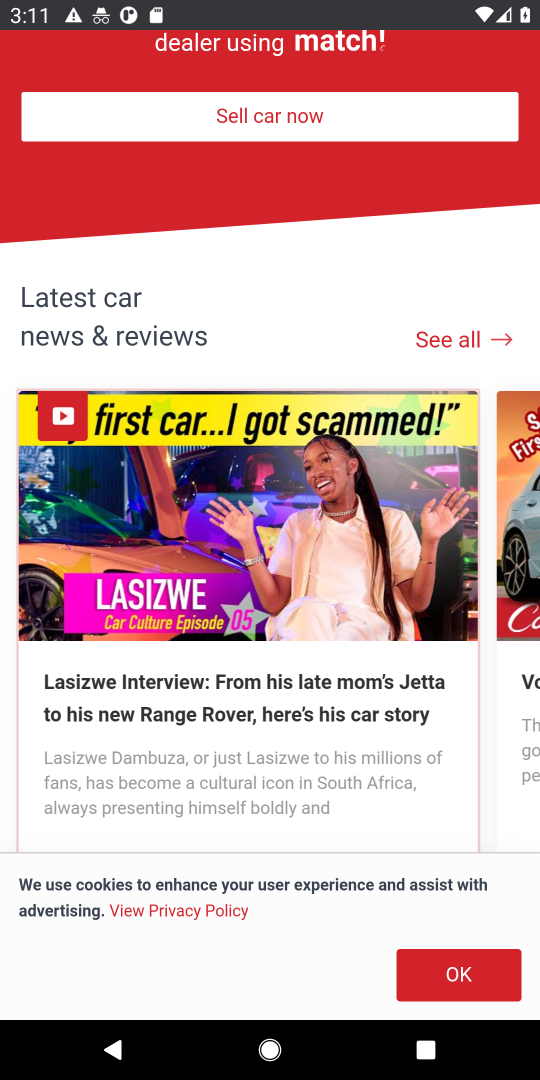
Step 99: drag from (417, 557) to (488, 192)
Your task to perform on an android device: Open a new incognito window in Chrome Image 100: 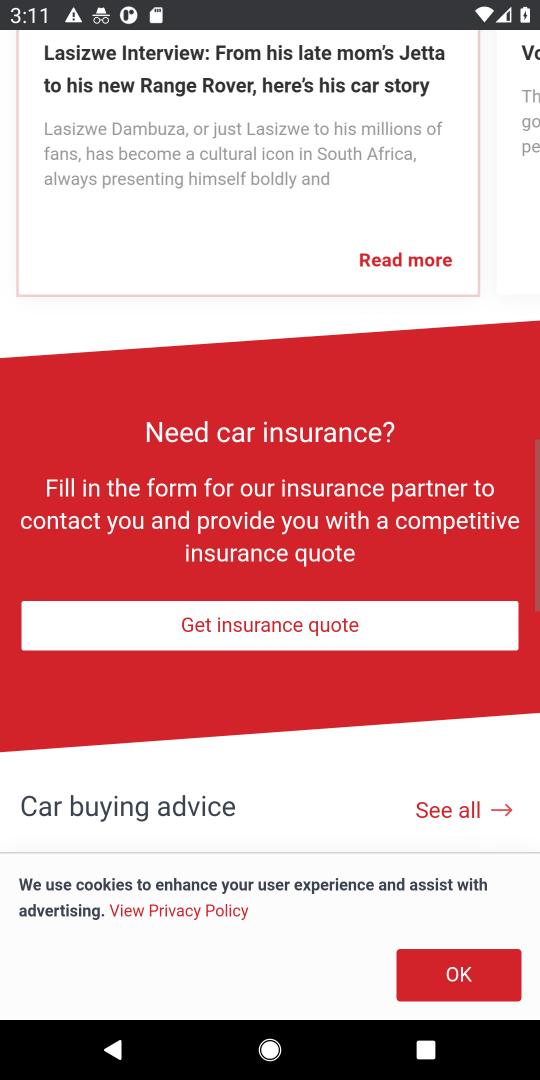
Step 100: press back button
Your task to perform on an android device: Open a new incognito window in Chrome Image 101: 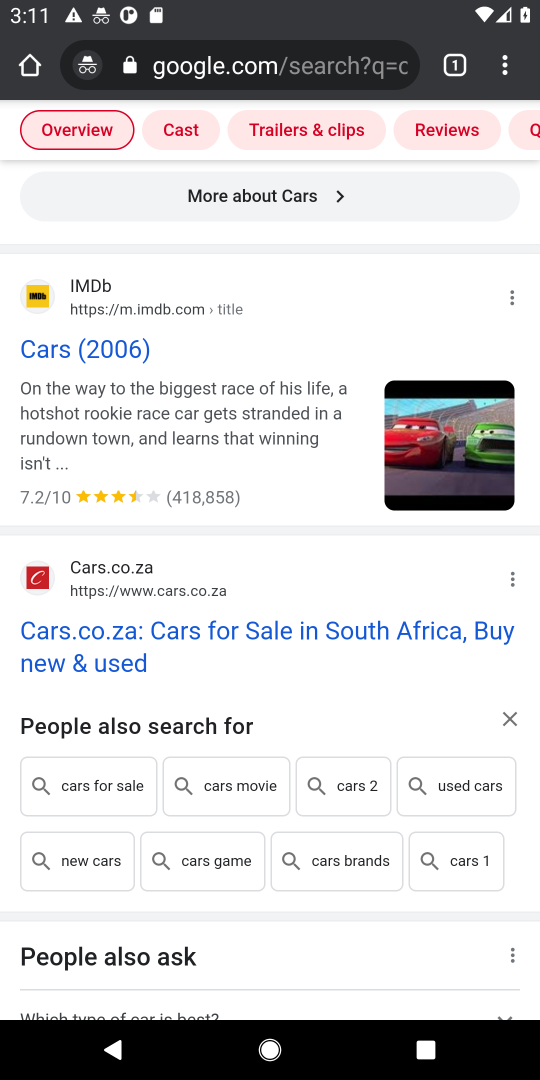
Step 101: drag from (379, 773) to (384, 661)
Your task to perform on an android device: Open a new incognito window in Chrome Image 102: 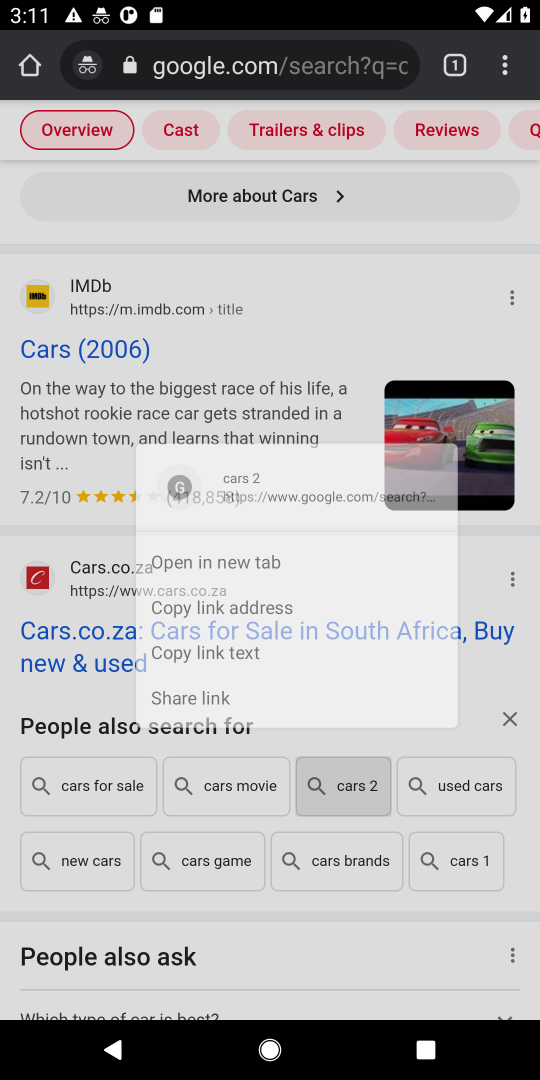
Step 102: click (380, 636)
Your task to perform on an android device: Open a new incognito window in Chrome Image 103: 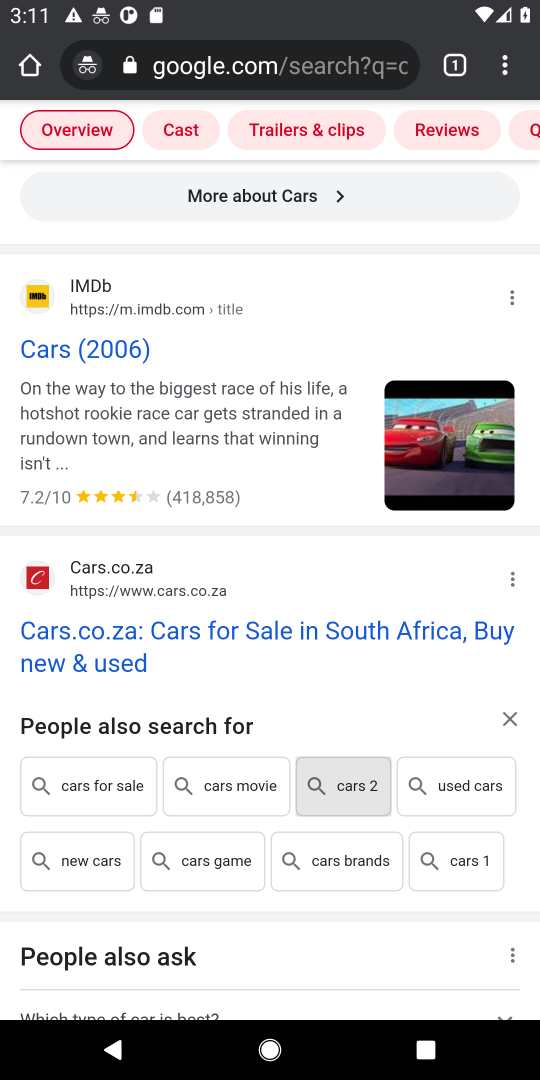
Step 103: click (347, 640)
Your task to perform on an android device: Open a new incognito window in Chrome Image 104: 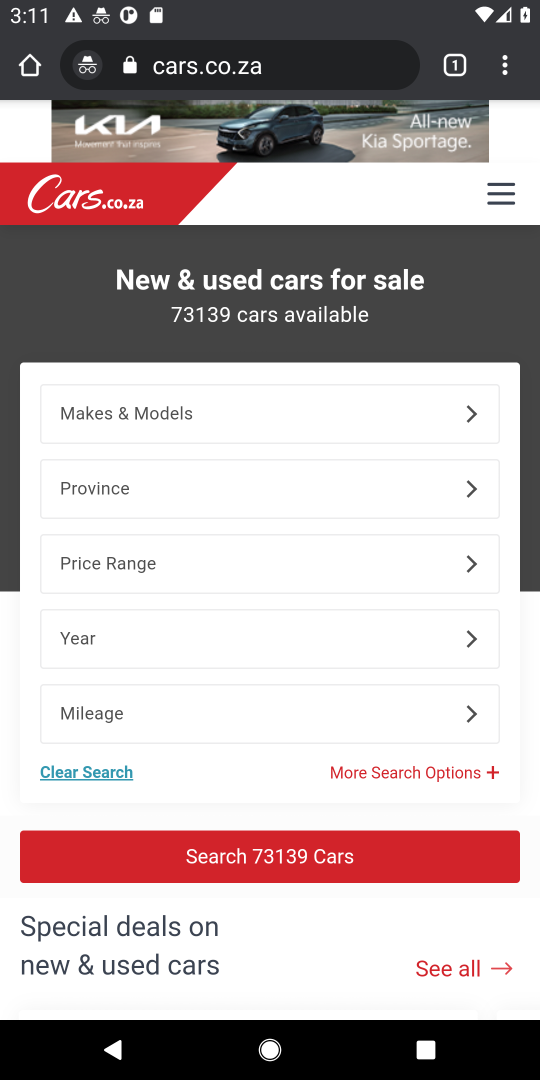
Step 104: drag from (368, 770) to (429, 185)
Your task to perform on an android device: Open a new incognito window in Chrome Image 105: 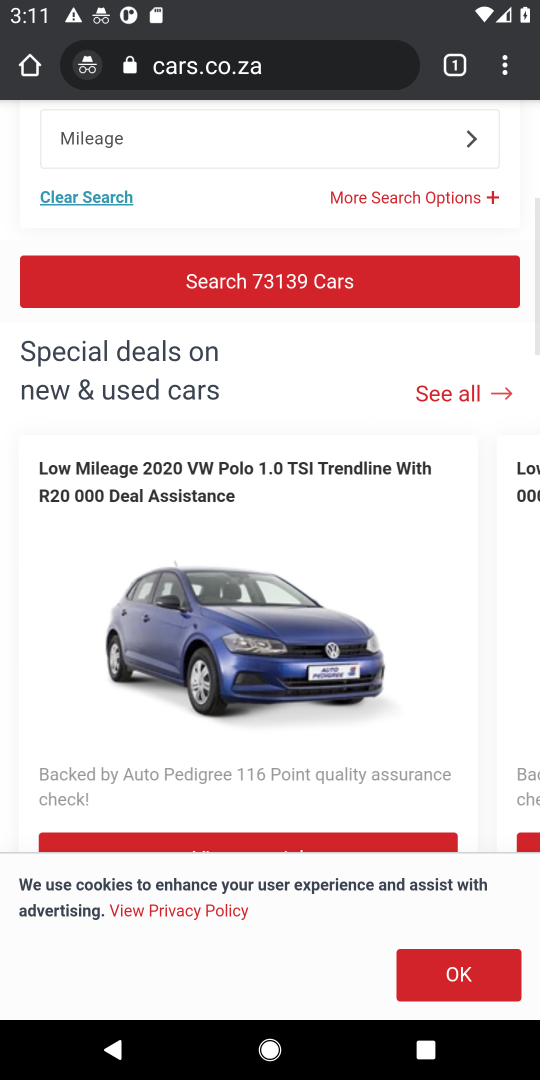
Step 105: drag from (331, 918) to (405, 272)
Your task to perform on an android device: Open a new incognito window in Chrome Image 106: 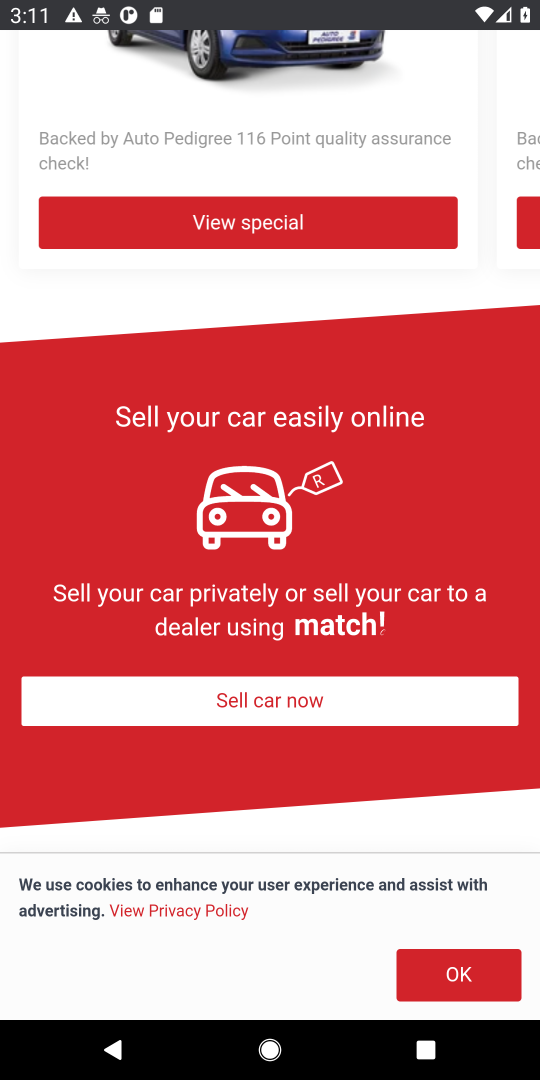
Step 106: drag from (475, 134) to (196, 116)
Your task to perform on an android device: Open a new incognito window in Chrome Image 107: 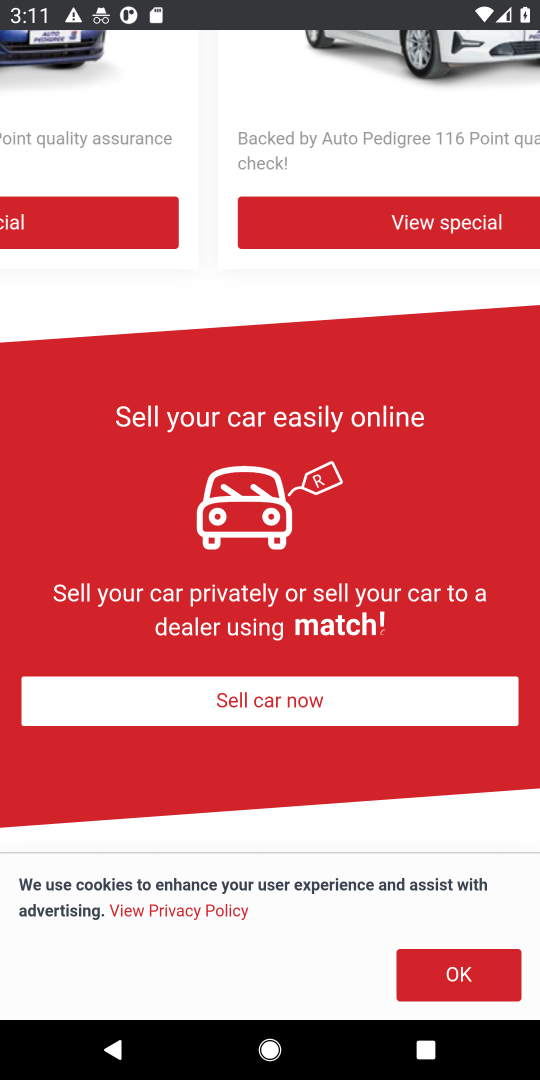
Step 107: drag from (447, 123) to (190, 125)
Your task to perform on an android device: Open a new incognito window in Chrome Image 108: 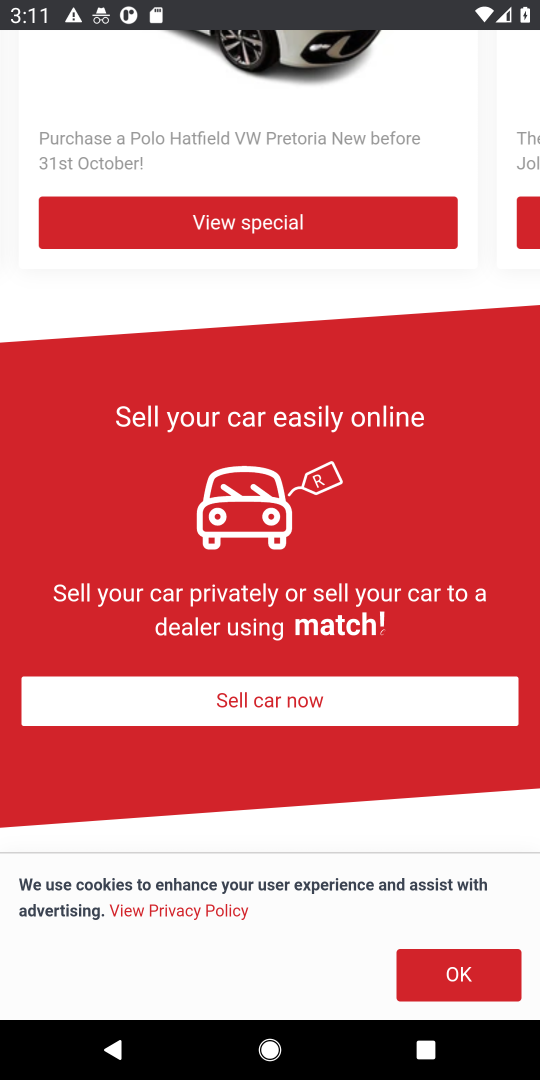
Step 108: drag from (480, 143) to (189, 151)
Your task to perform on an android device: Open a new incognito window in Chrome Image 109: 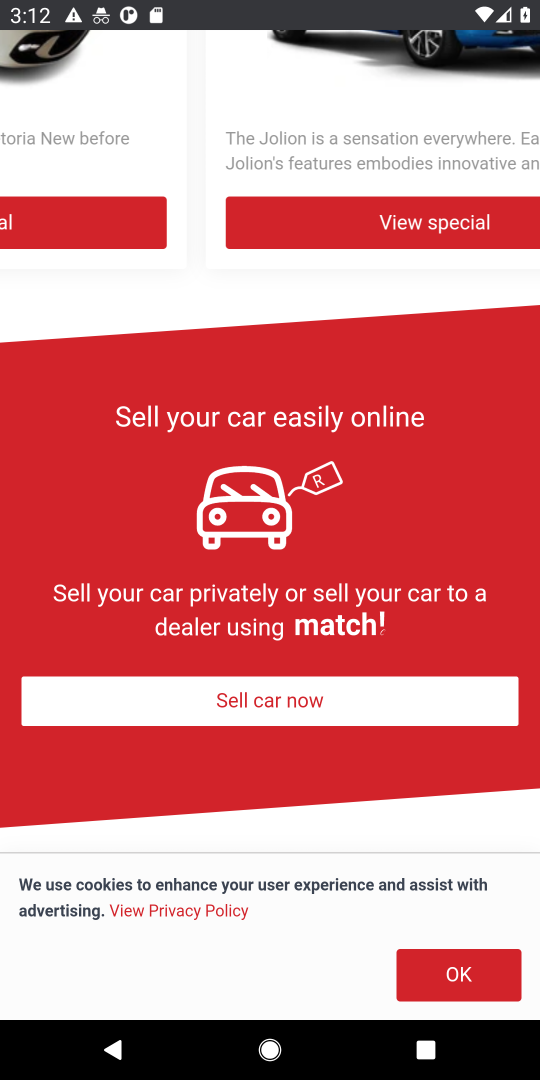
Step 109: click (274, 138)
Your task to perform on an android device: Open a new incognito window in Chrome Image 110: 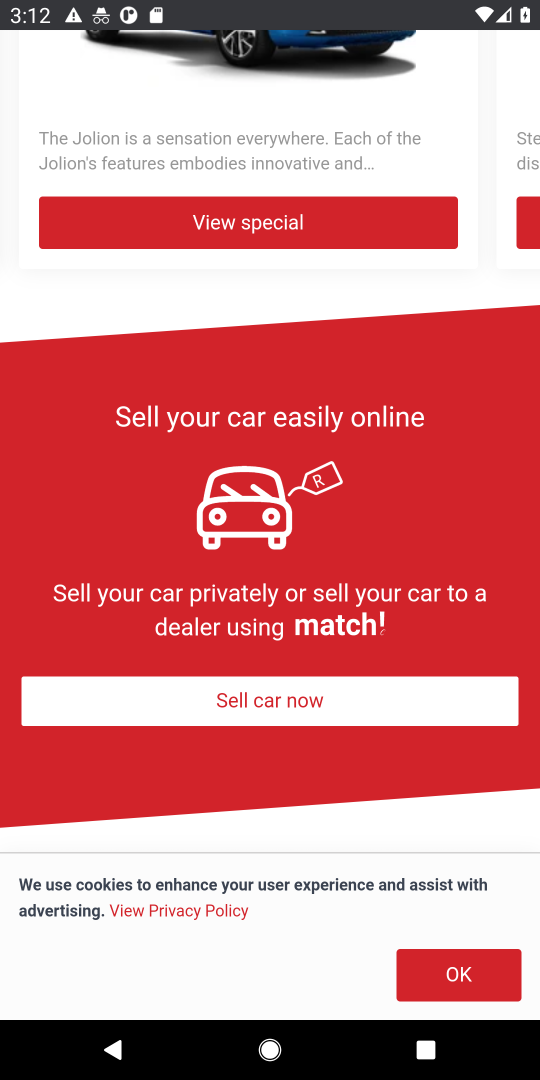
Step 110: press back button
Your task to perform on an android device: Open a new incognito window in Chrome Image 111: 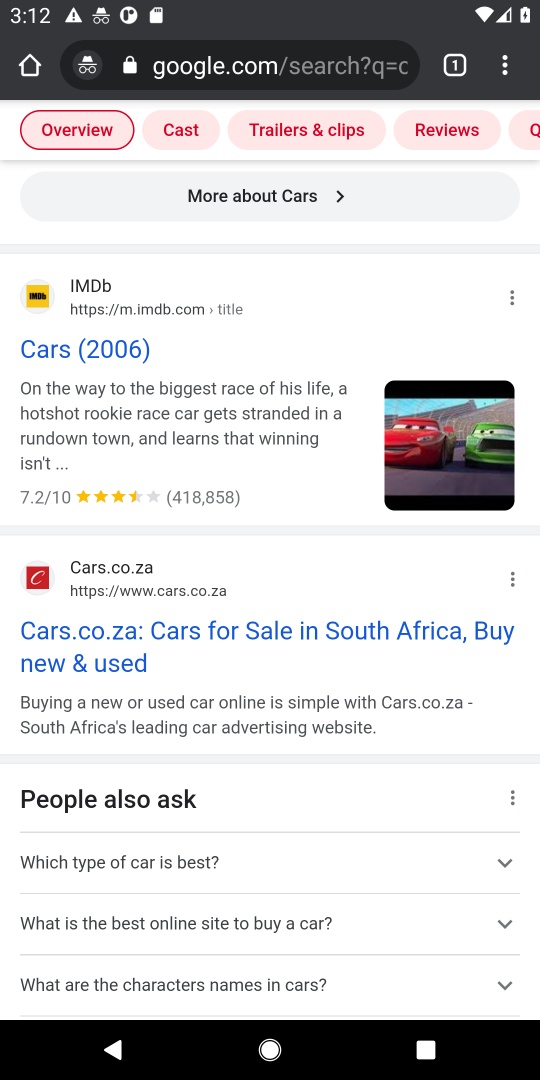
Step 111: drag from (318, 833) to (385, 268)
Your task to perform on an android device: Open a new incognito window in Chrome Image 112: 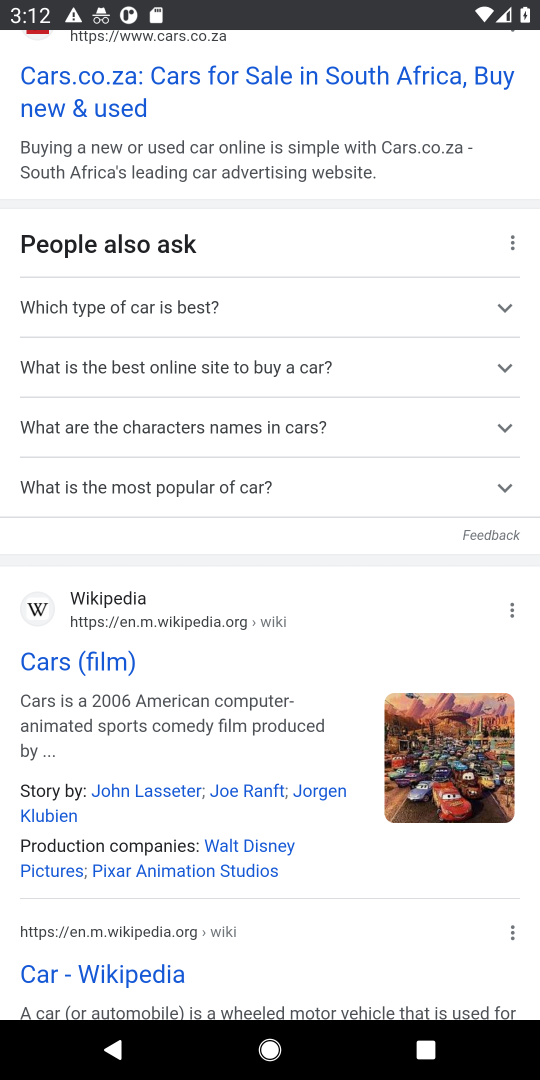
Step 112: click (93, 650)
Your task to perform on an android device: Open a new incognito window in Chrome Image 113: 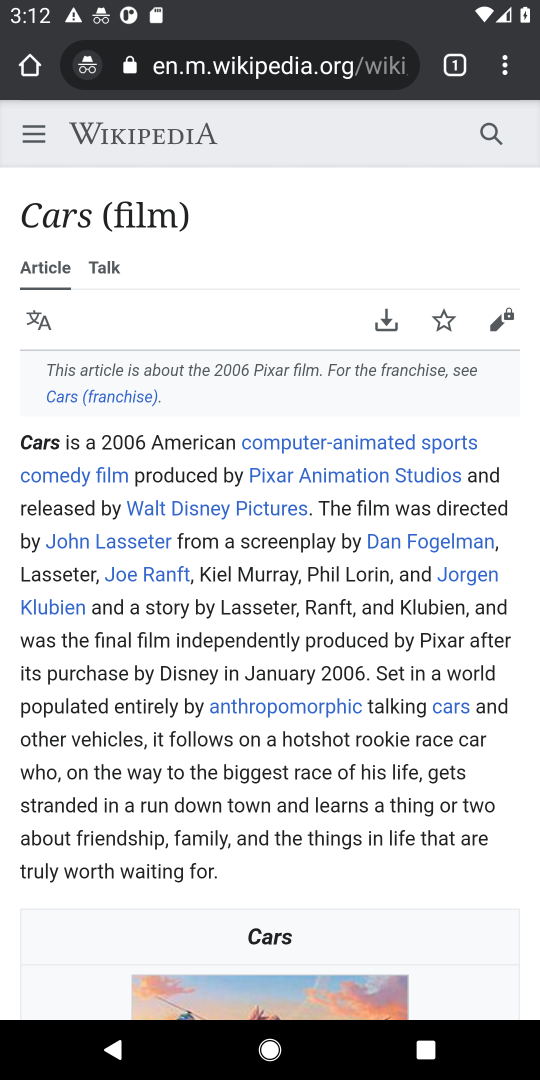
Step 113: task complete